Your task to perform on an android device: open app "The Home Depot" (install if not already installed) Image 0: 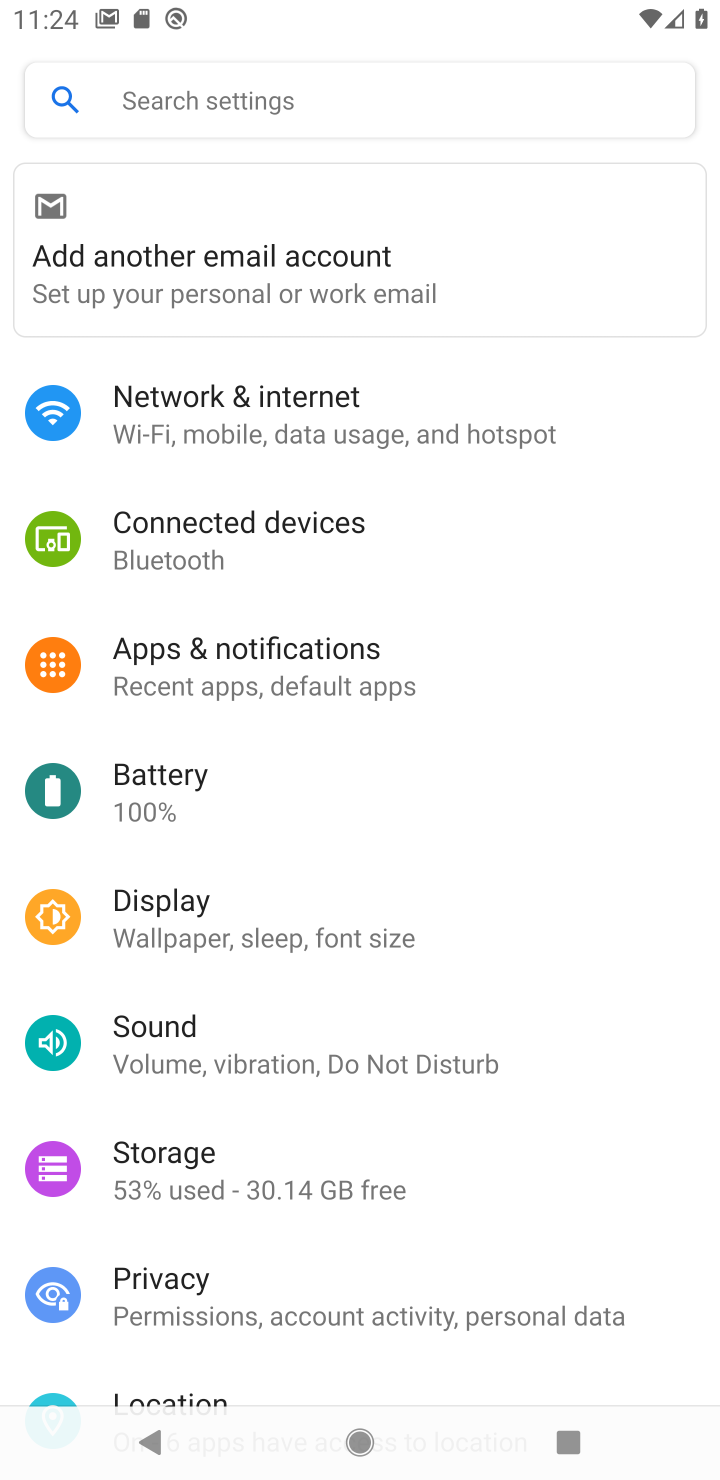
Step 0: press back button
Your task to perform on an android device: open app "The Home Depot" (install if not already installed) Image 1: 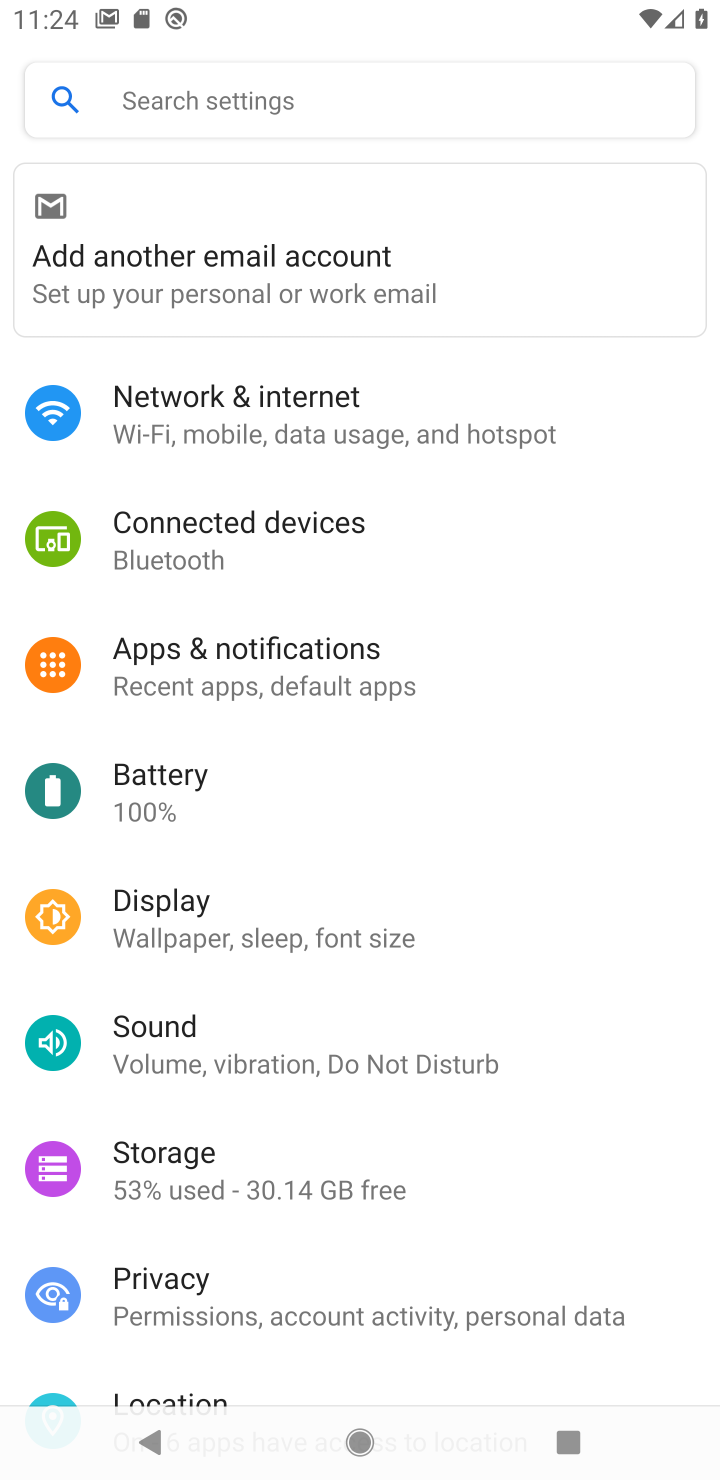
Step 1: press back button
Your task to perform on an android device: open app "The Home Depot" (install if not already installed) Image 2: 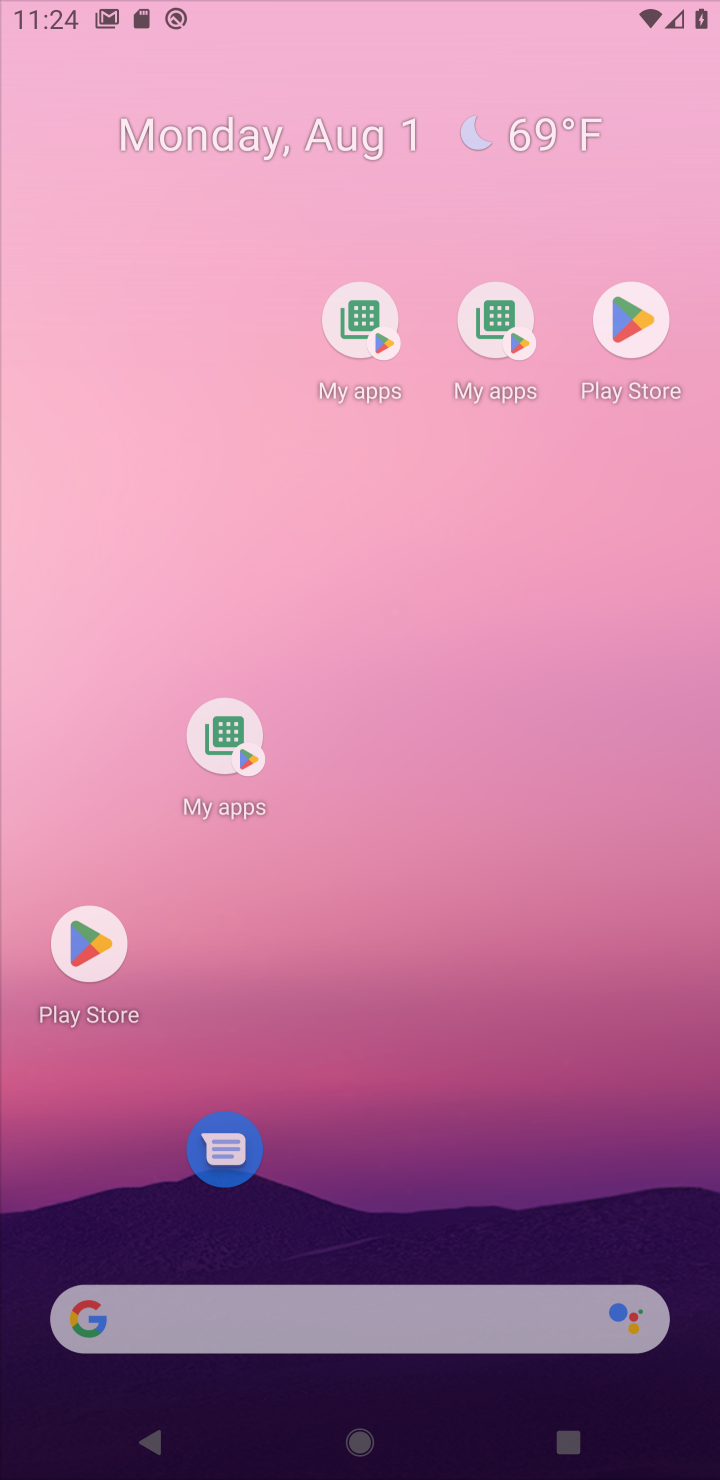
Step 2: press home button
Your task to perform on an android device: open app "The Home Depot" (install if not already installed) Image 3: 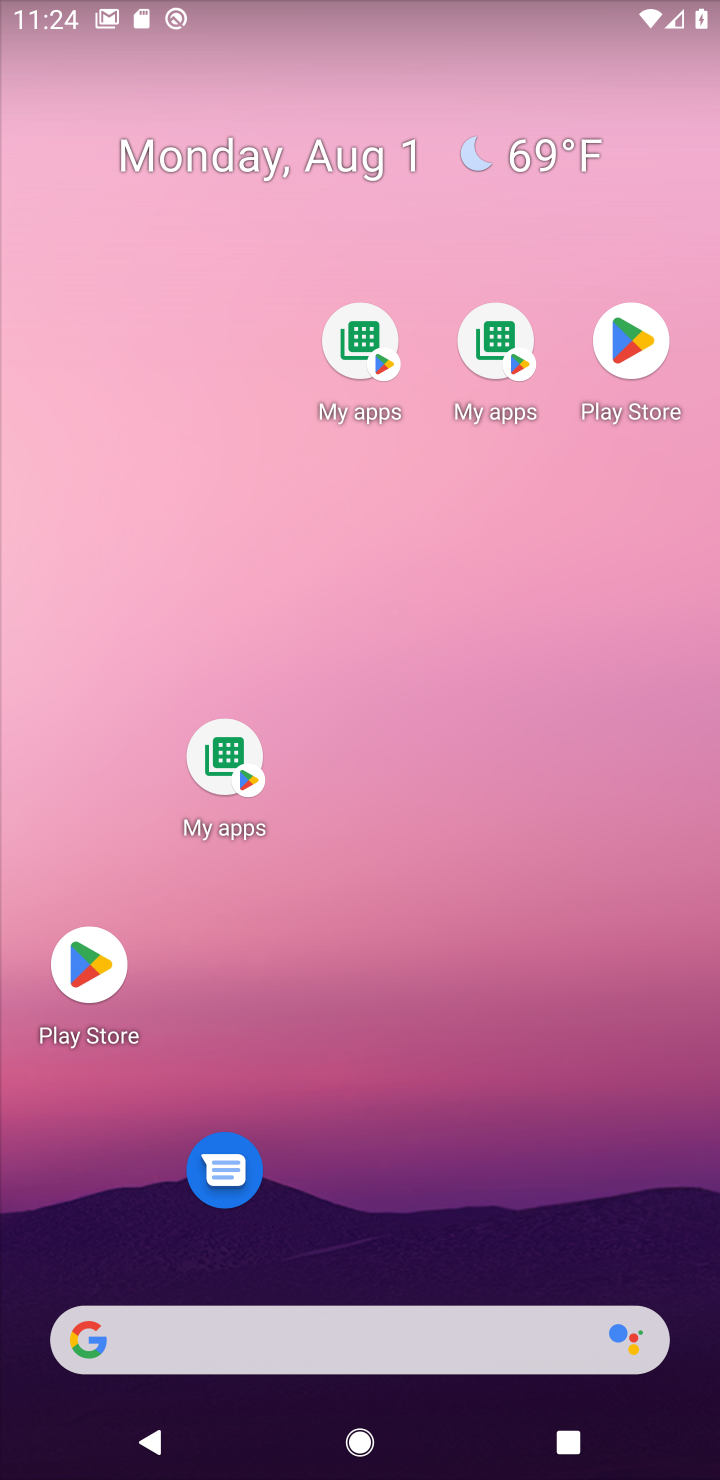
Step 3: click (639, 337)
Your task to perform on an android device: open app "The Home Depot" (install if not already installed) Image 4: 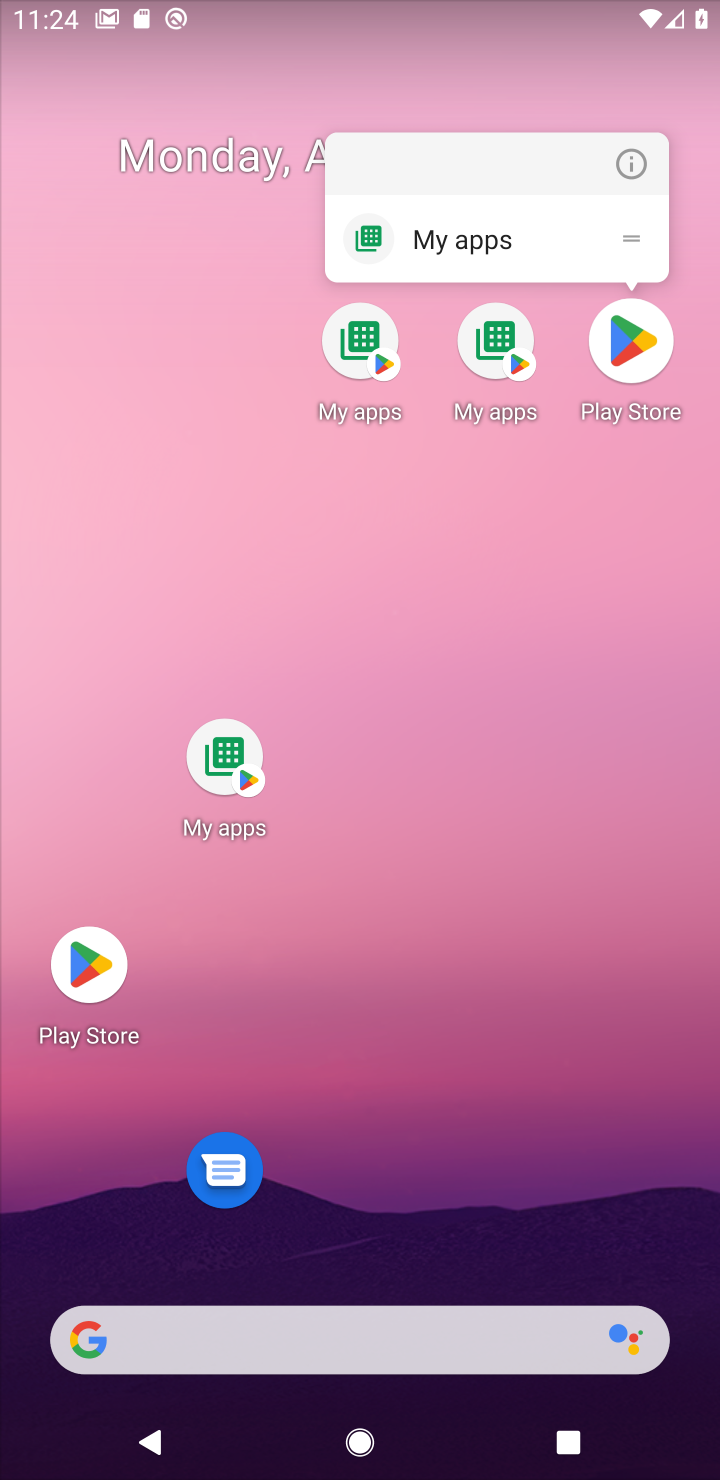
Step 4: click (639, 337)
Your task to perform on an android device: open app "The Home Depot" (install if not already installed) Image 5: 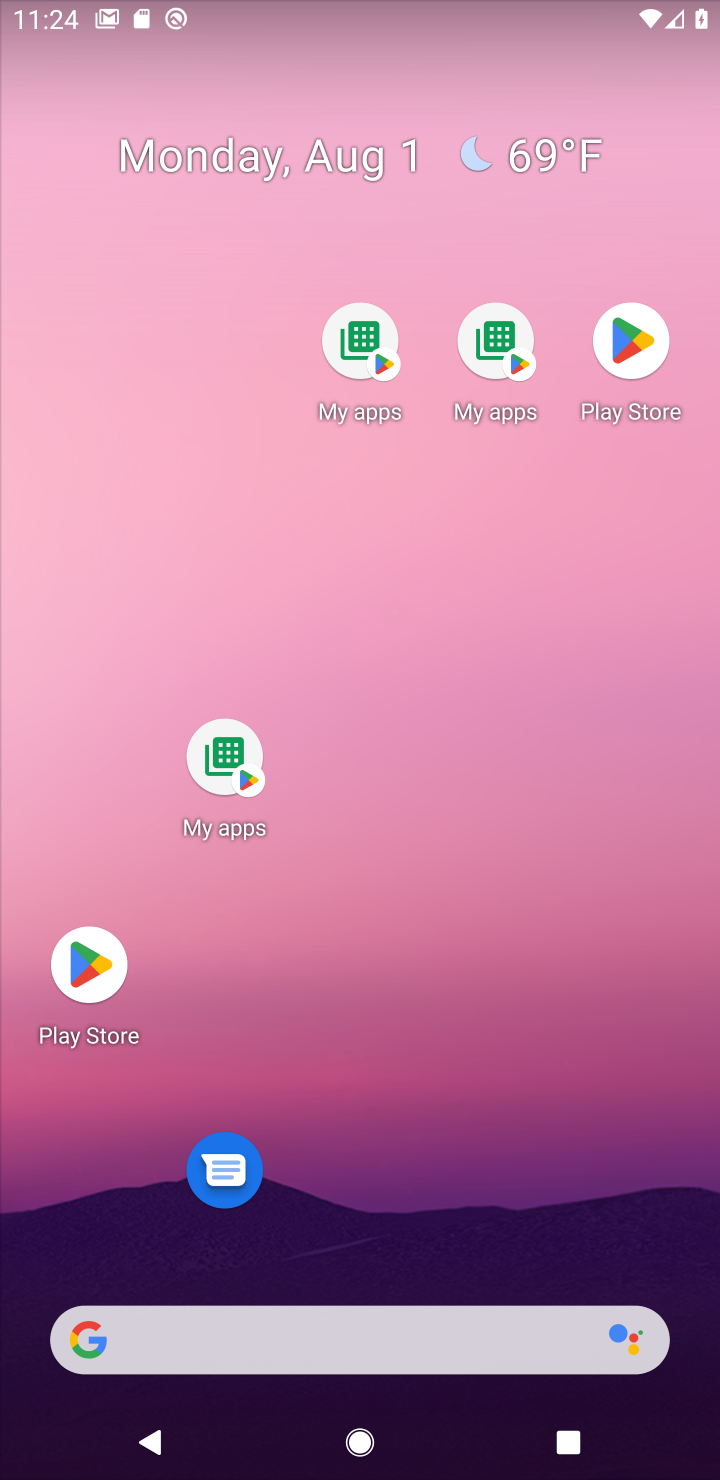
Step 5: click (439, 235)
Your task to perform on an android device: open app "The Home Depot" (install if not already installed) Image 6: 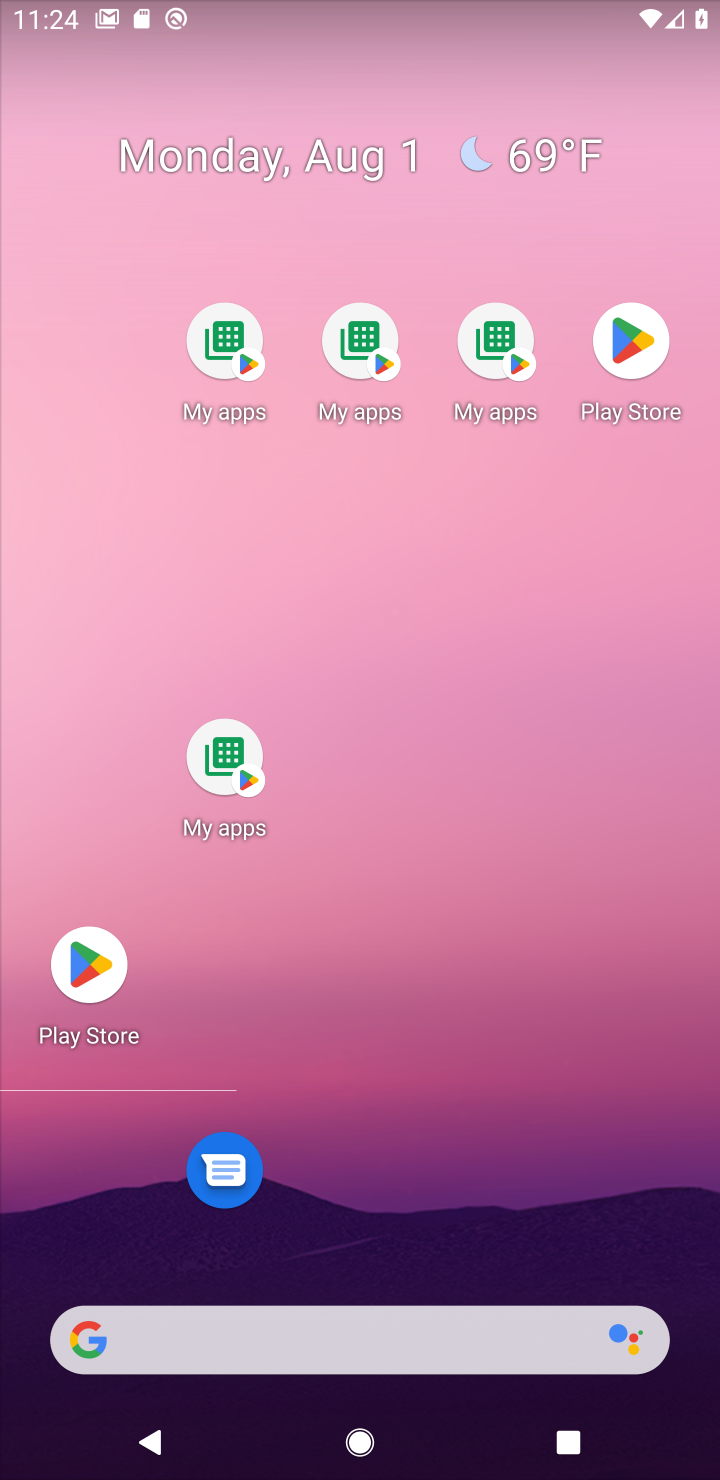
Step 6: click (474, 249)
Your task to perform on an android device: open app "The Home Depot" (install if not already installed) Image 7: 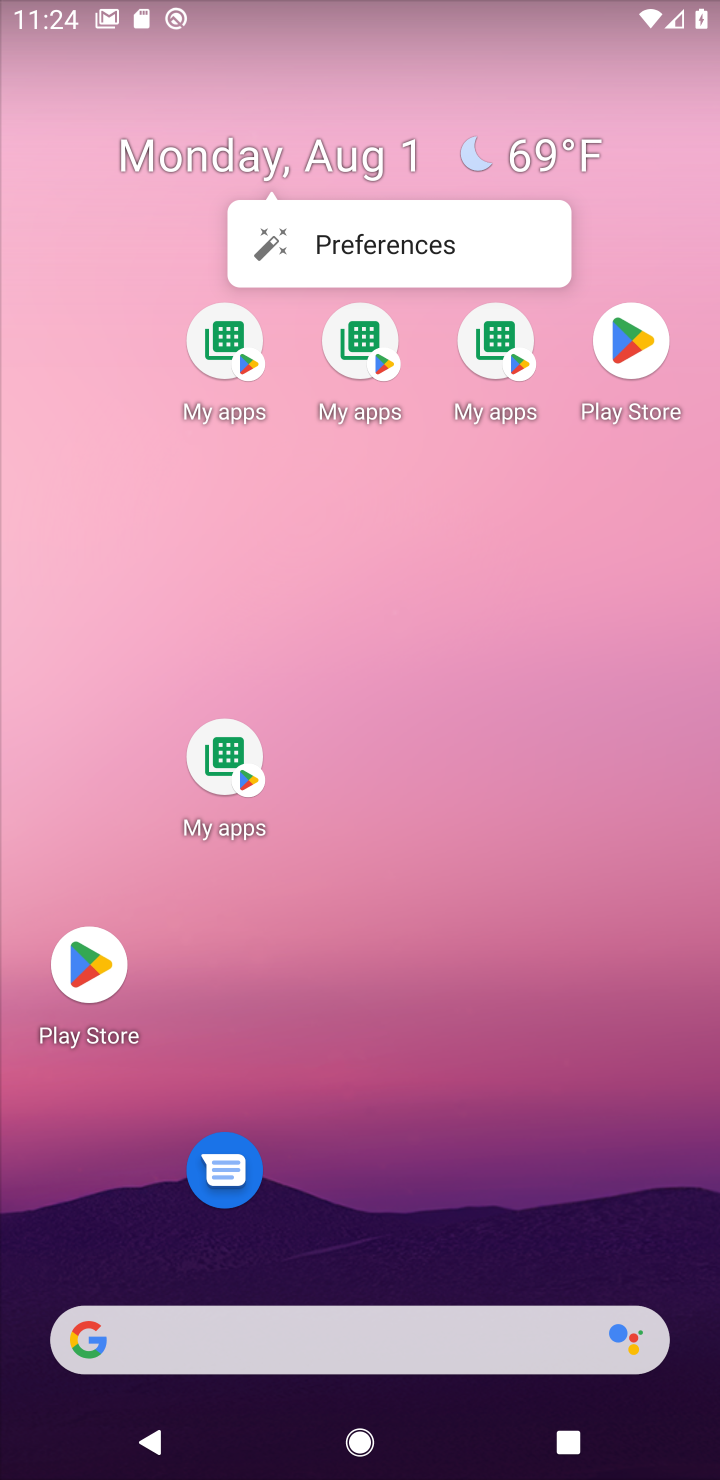
Step 7: click (636, 340)
Your task to perform on an android device: open app "The Home Depot" (install if not already installed) Image 8: 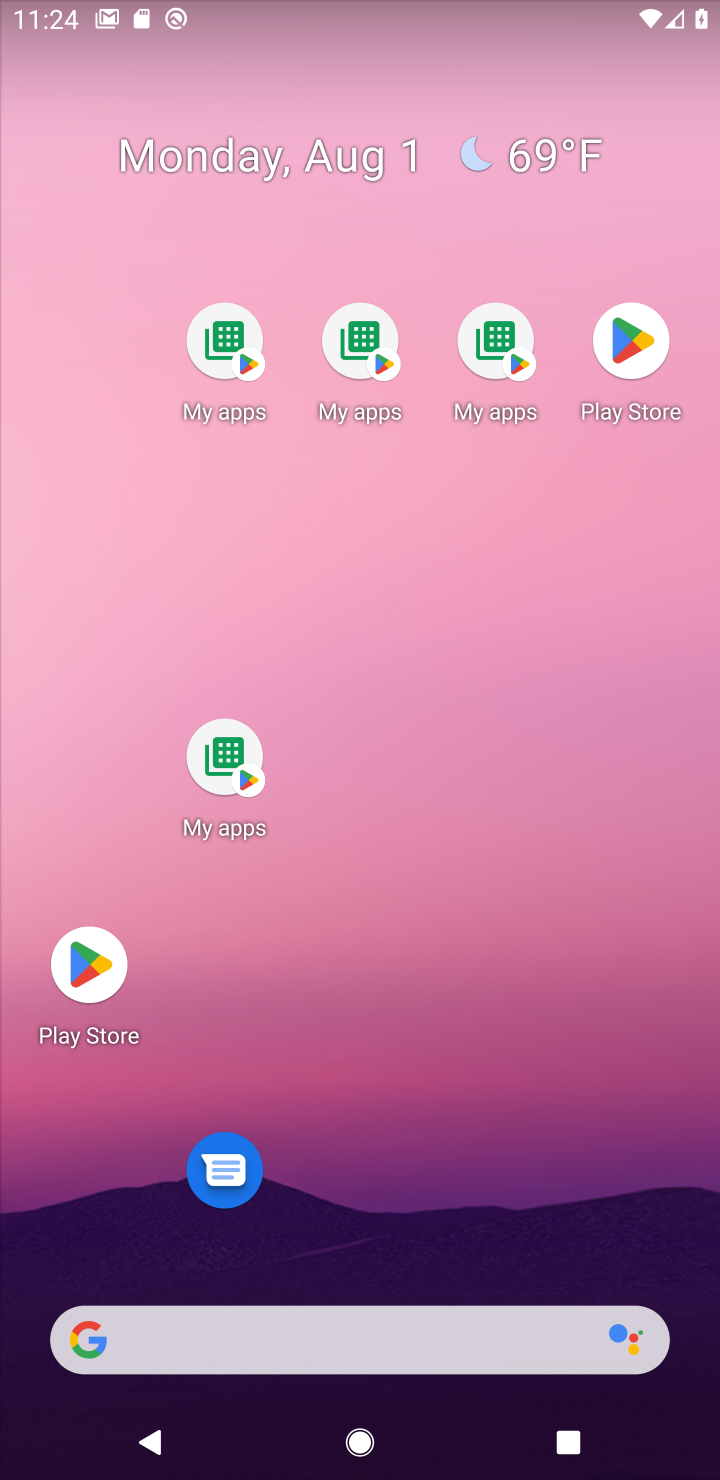
Step 8: click (614, 317)
Your task to perform on an android device: open app "The Home Depot" (install if not already installed) Image 9: 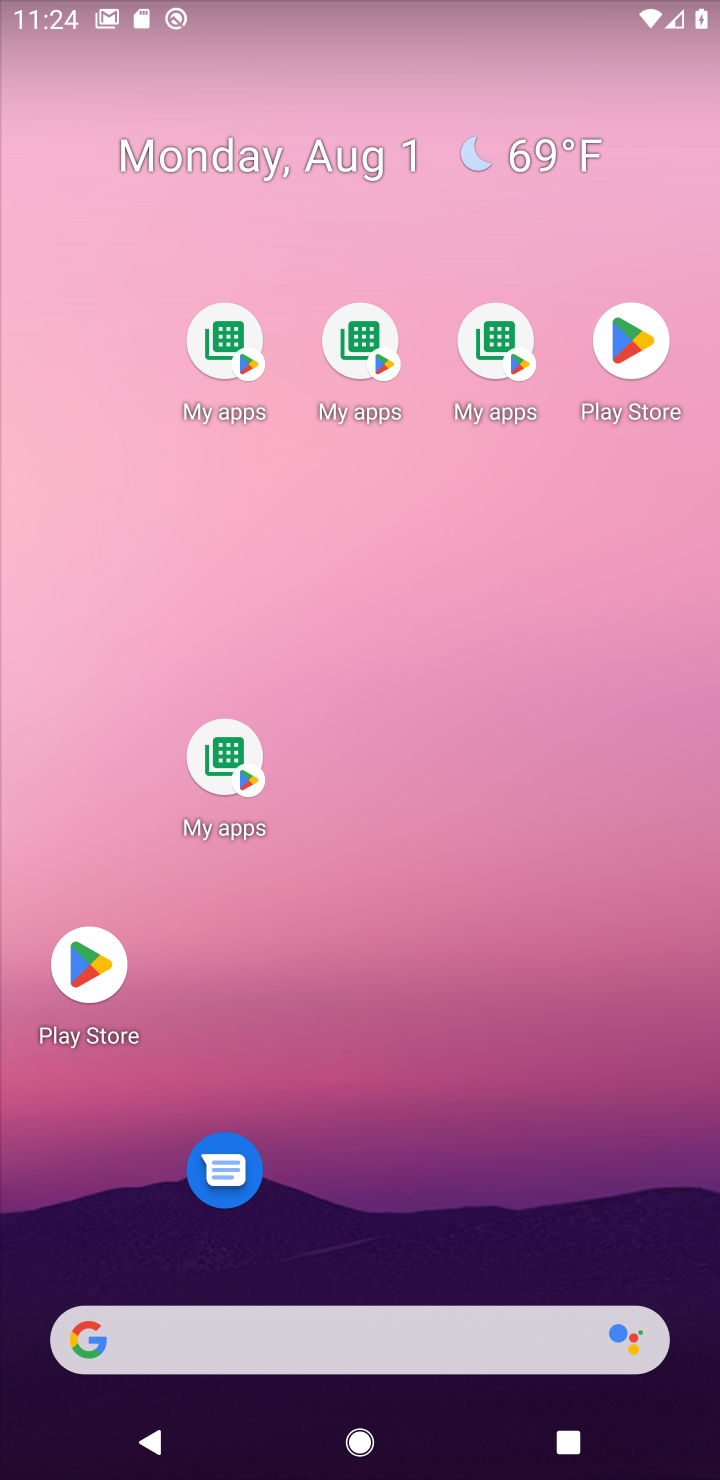
Step 9: click (613, 323)
Your task to perform on an android device: open app "The Home Depot" (install if not already installed) Image 10: 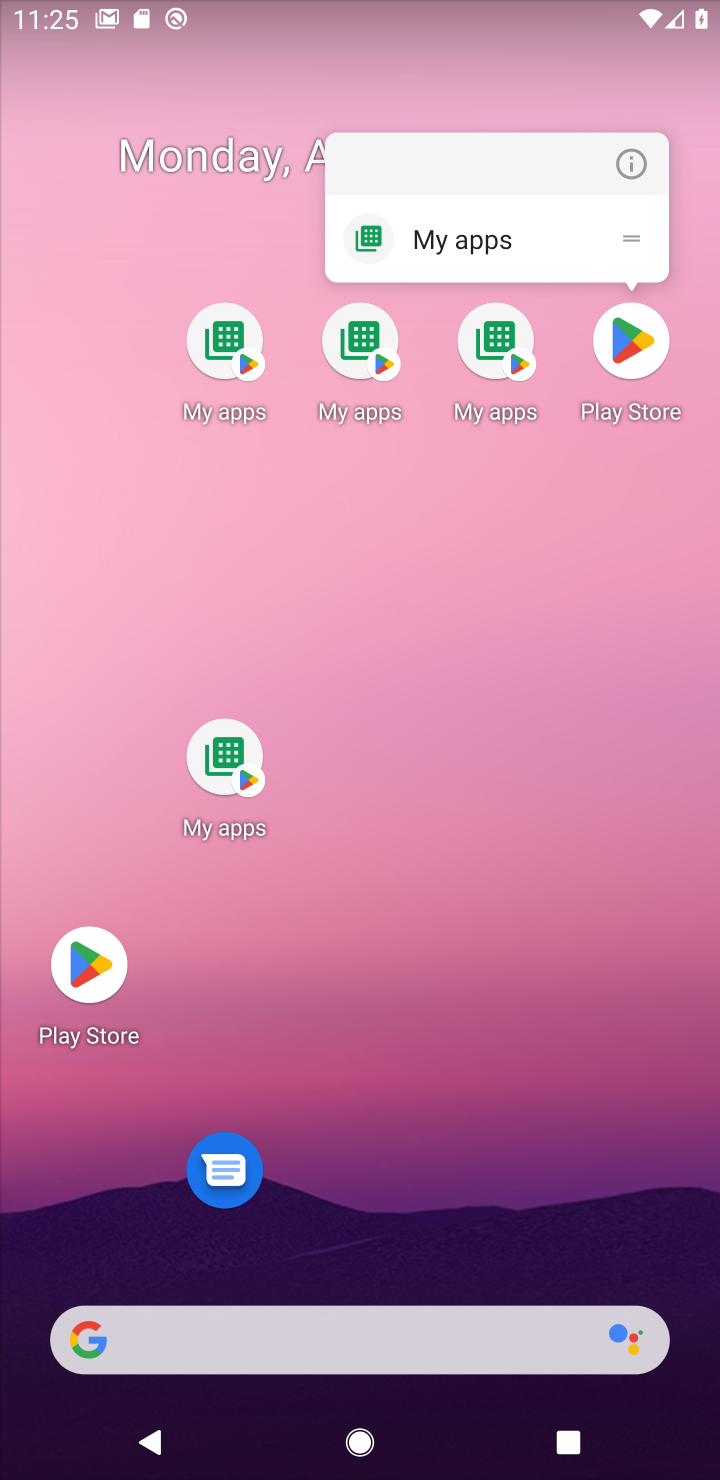
Step 10: click (386, 213)
Your task to perform on an android device: open app "The Home Depot" (install if not already installed) Image 11: 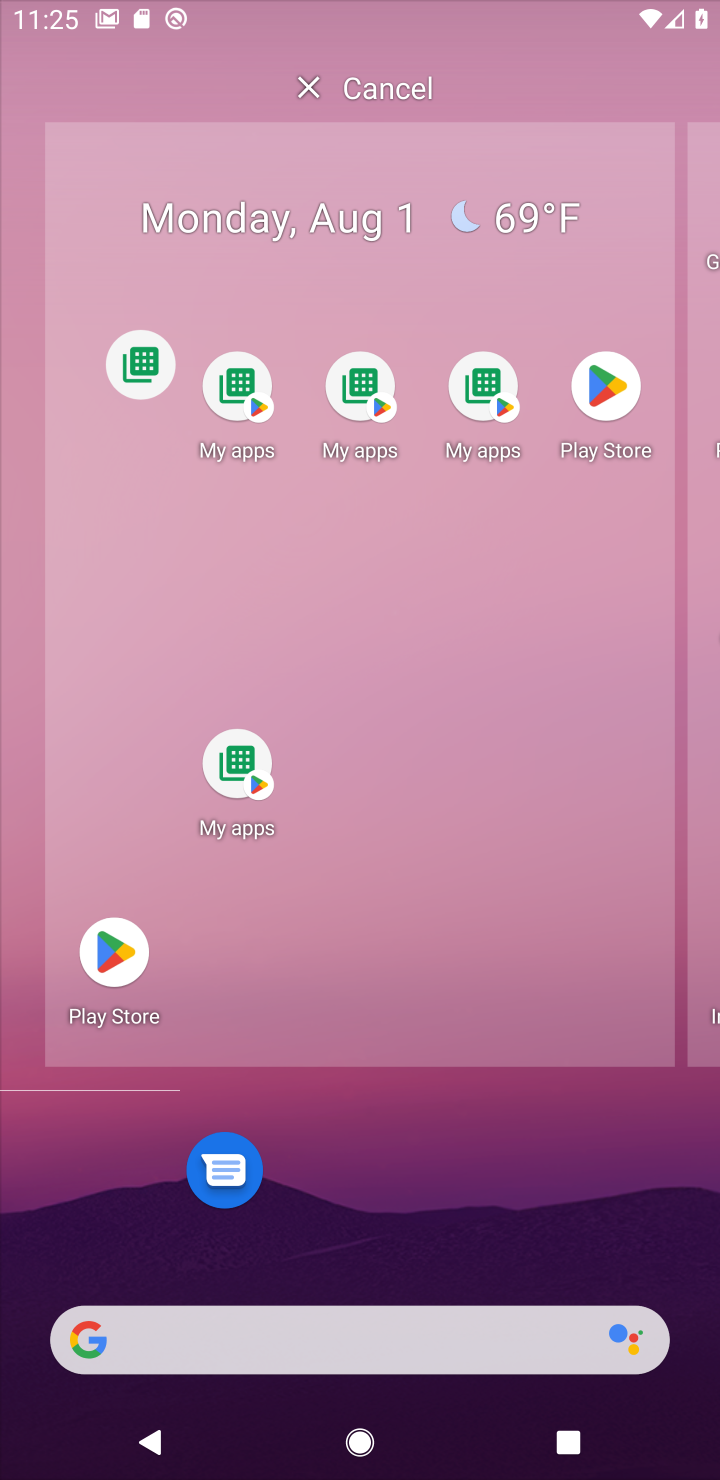
Step 11: click (488, 253)
Your task to perform on an android device: open app "The Home Depot" (install if not already installed) Image 12: 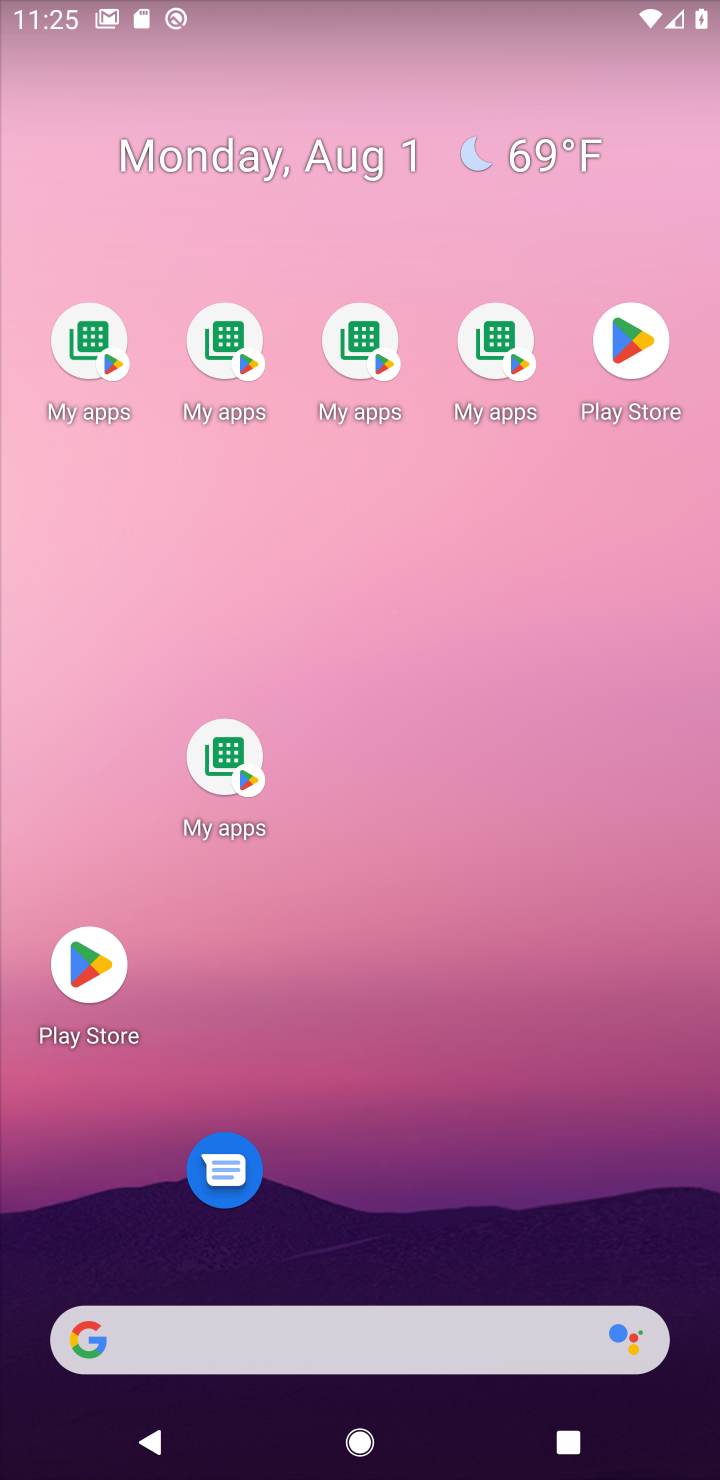
Step 12: drag from (350, 145) to (454, 337)
Your task to perform on an android device: open app "The Home Depot" (install if not already installed) Image 13: 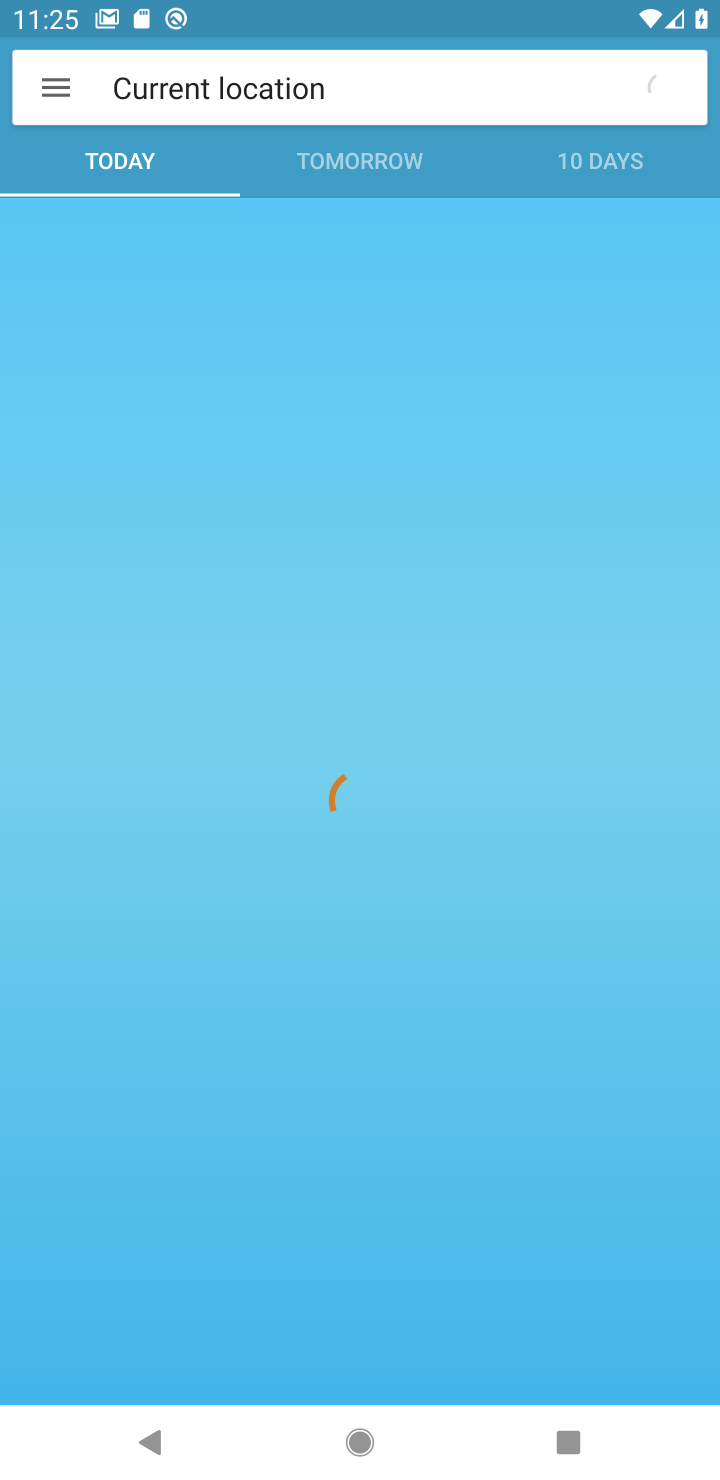
Step 13: drag from (146, 693) to (173, 238)
Your task to perform on an android device: open app "The Home Depot" (install if not already installed) Image 14: 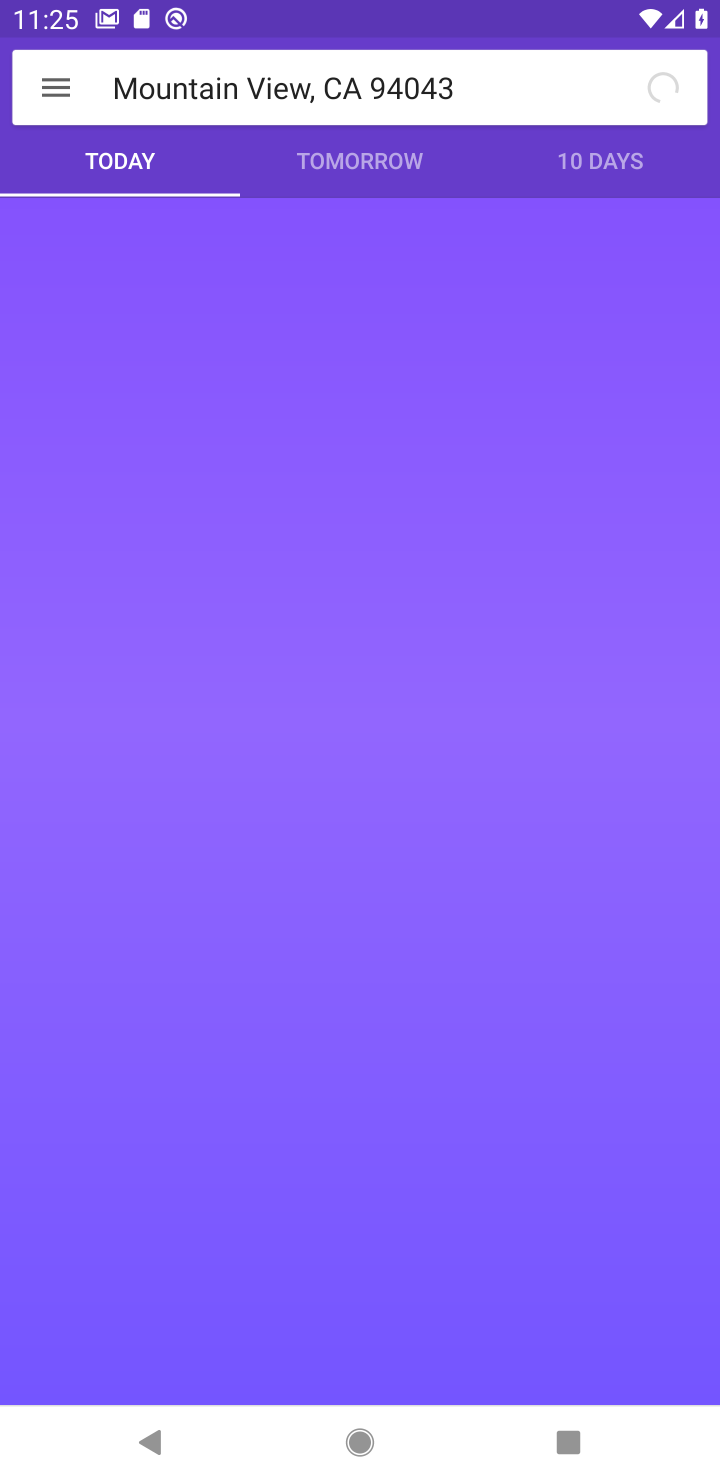
Step 14: press back button
Your task to perform on an android device: open app "The Home Depot" (install if not already installed) Image 15: 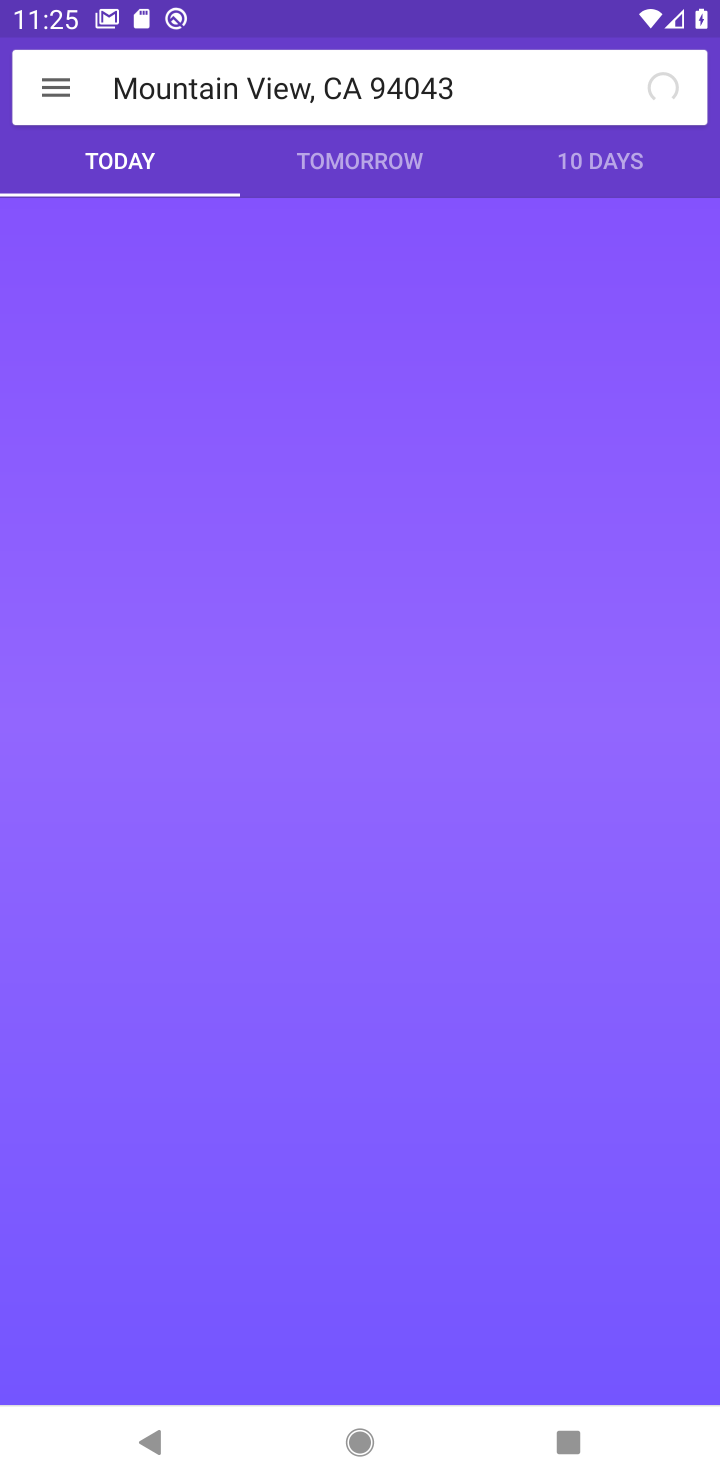
Step 15: drag from (227, 51) to (431, 190)
Your task to perform on an android device: open app "The Home Depot" (install if not already installed) Image 16: 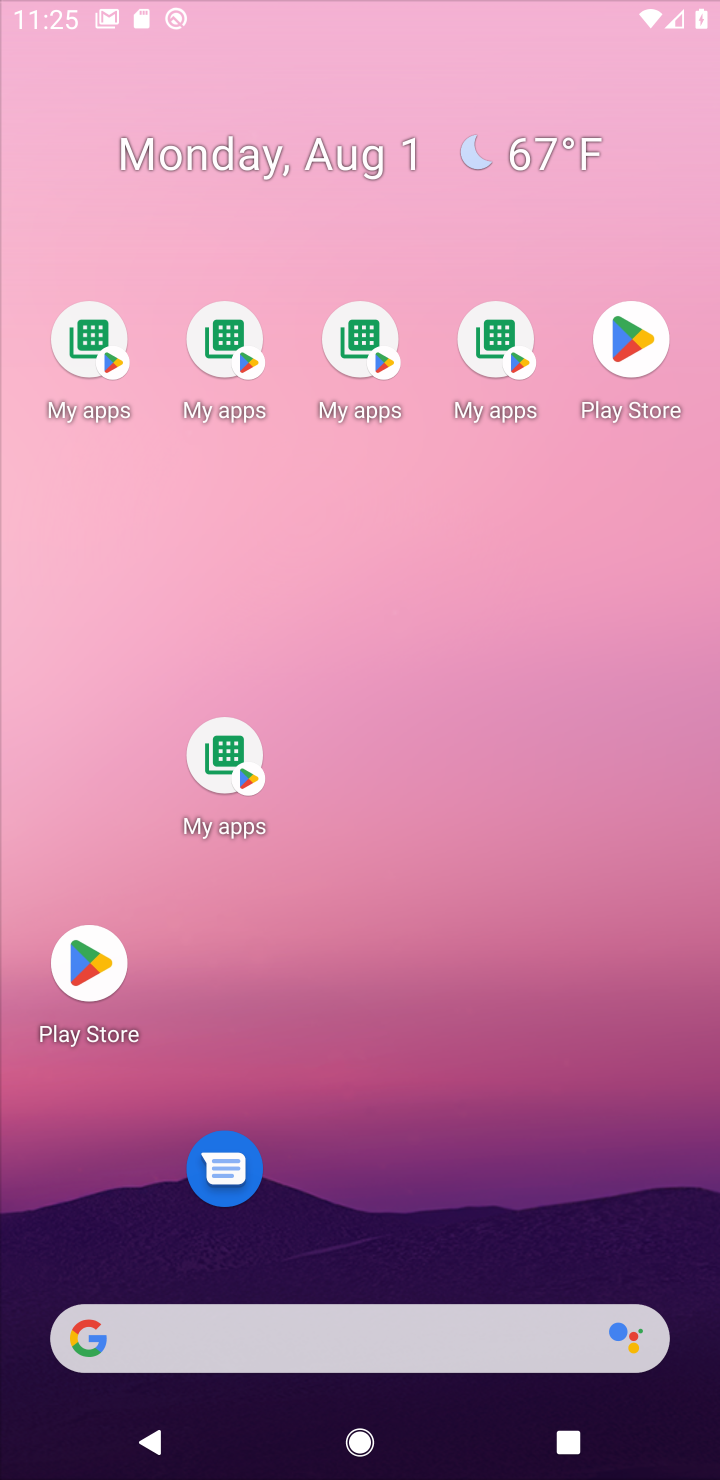
Step 16: press home button
Your task to perform on an android device: open app "The Home Depot" (install if not already installed) Image 17: 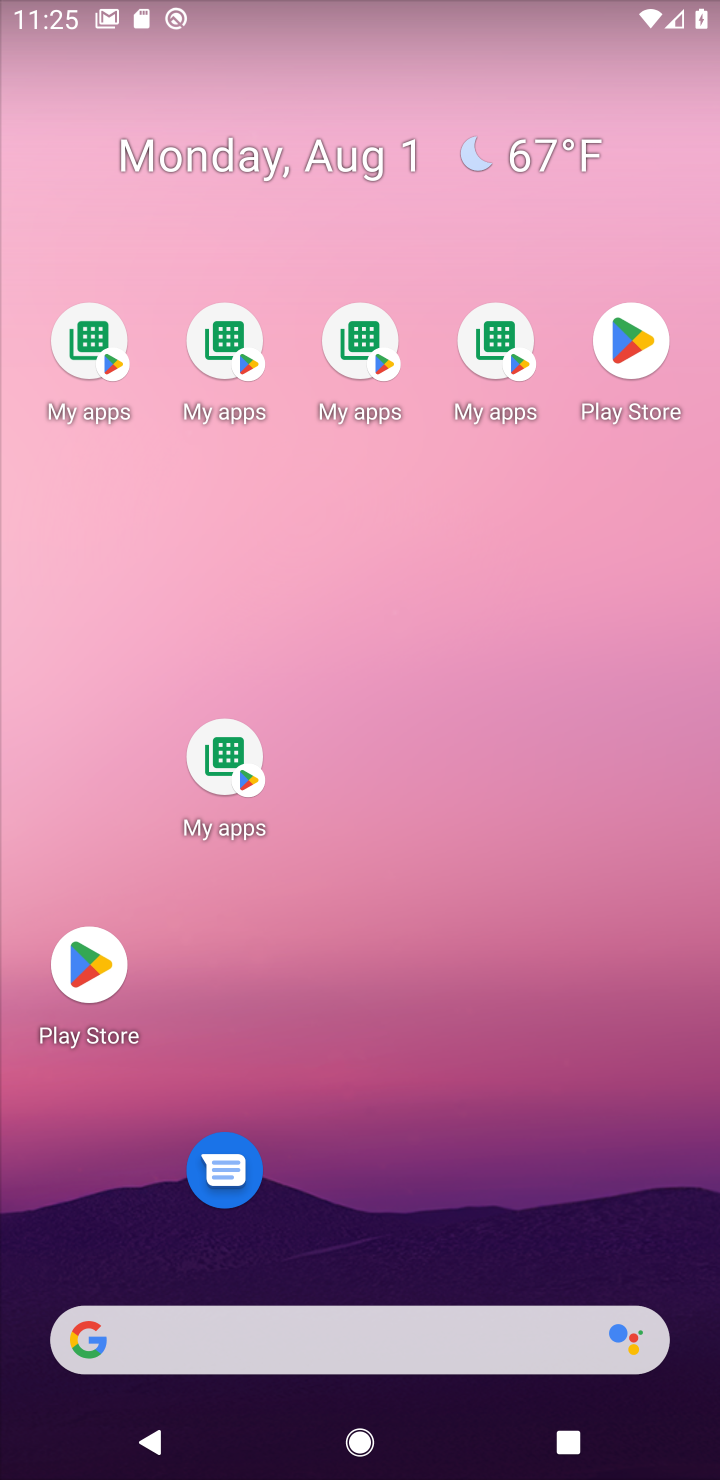
Step 17: click (360, 524)
Your task to perform on an android device: open app "The Home Depot" (install if not already installed) Image 18: 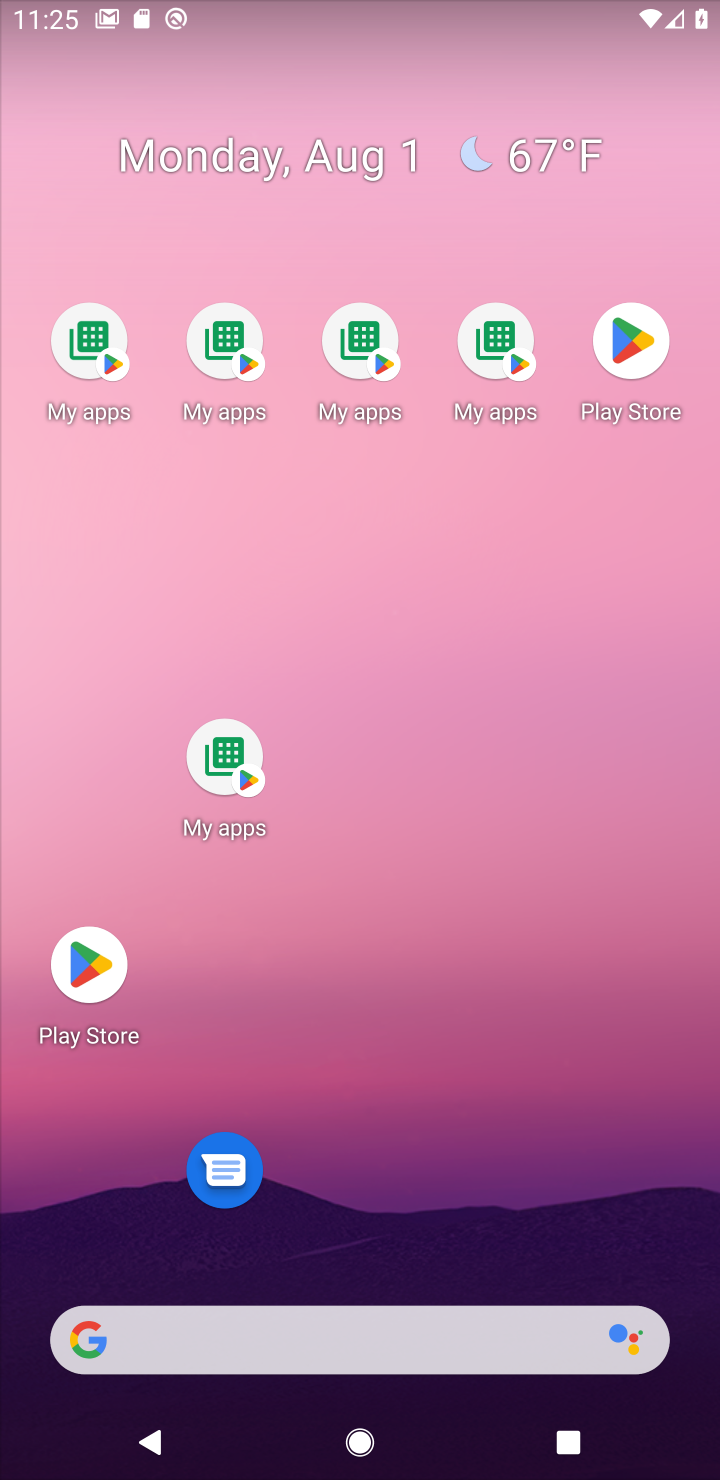
Step 18: drag from (404, 463) to (454, 138)
Your task to perform on an android device: open app "The Home Depot" (install if not already installed) Image 19: 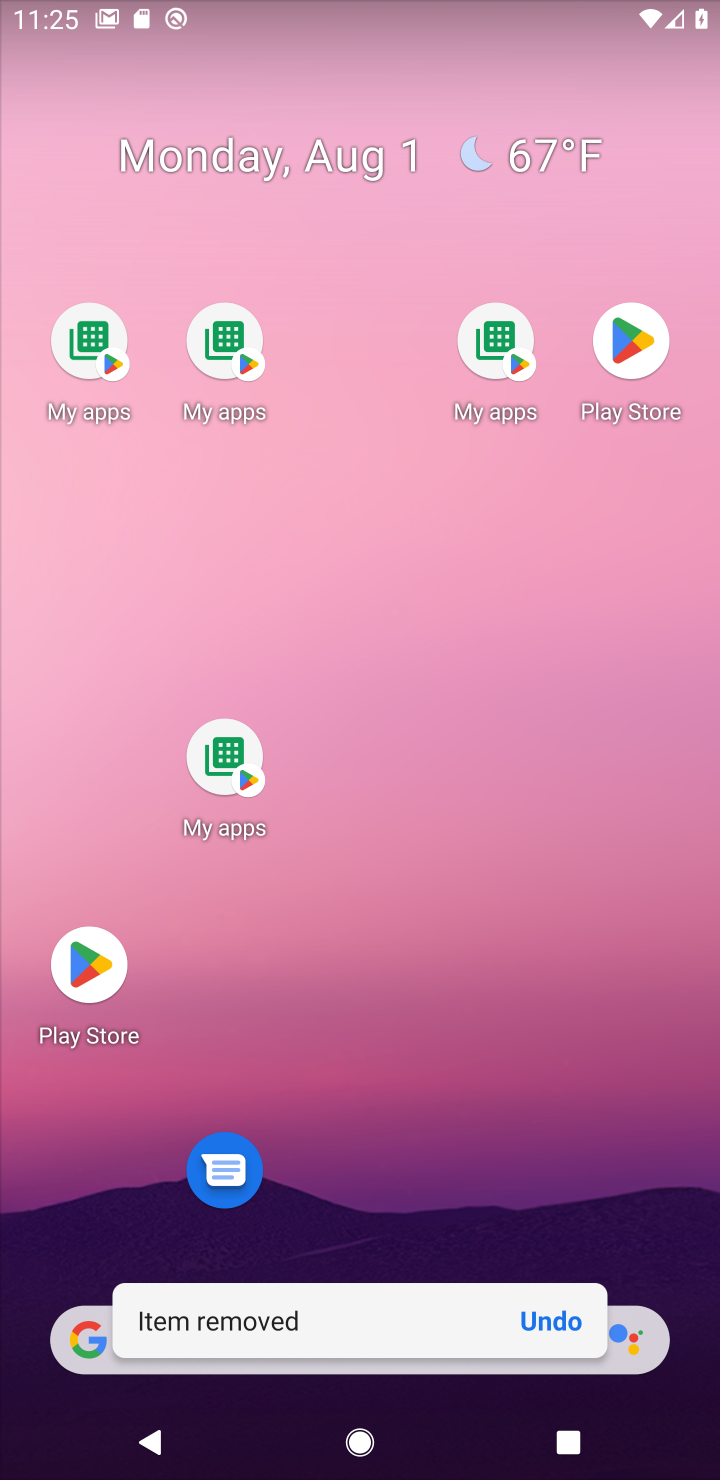
Step 19: click (79, 960)
Your task to perform on an android device: open app "The Home Depot" (install if not already installed) Image 20: 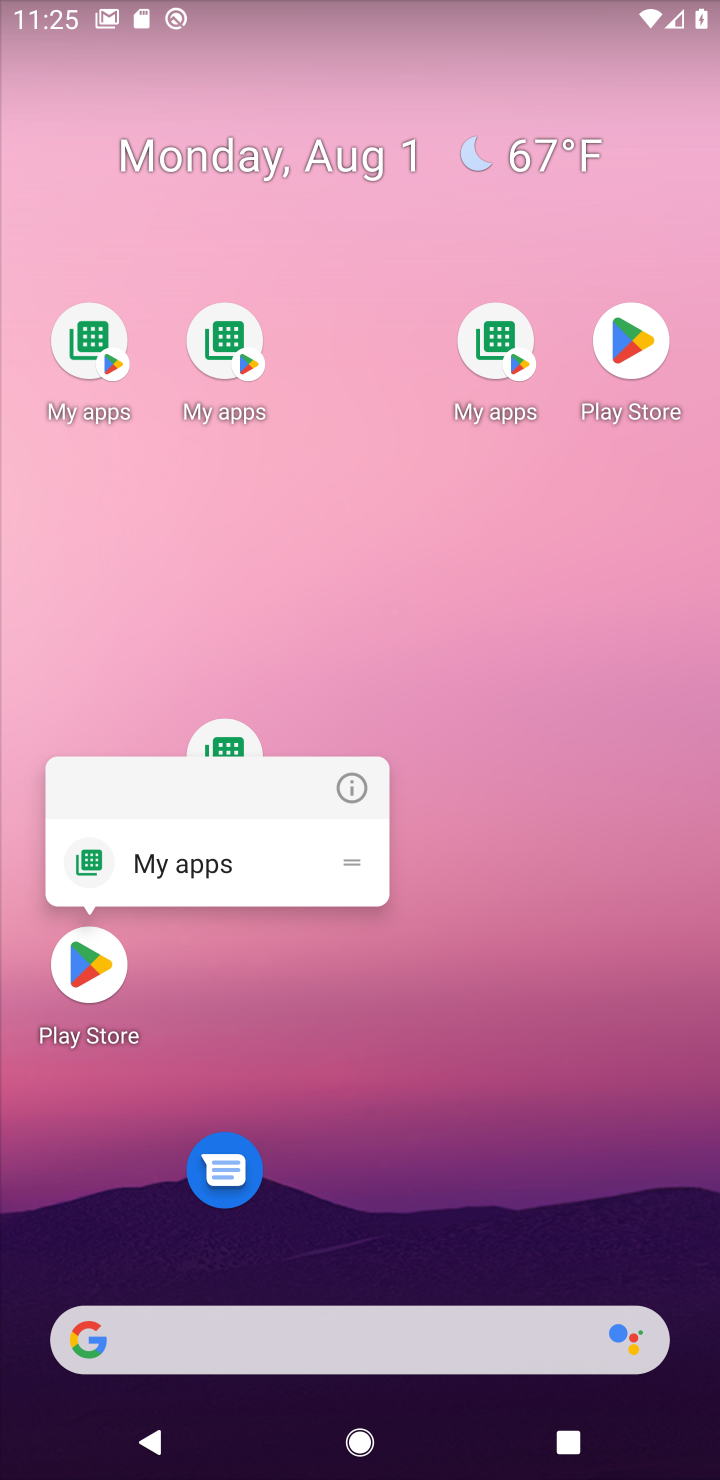
Step 20: click (111, 982)
Your task to perform on an android device: open app "The Home Depot" (install if not already installed) Image 21: 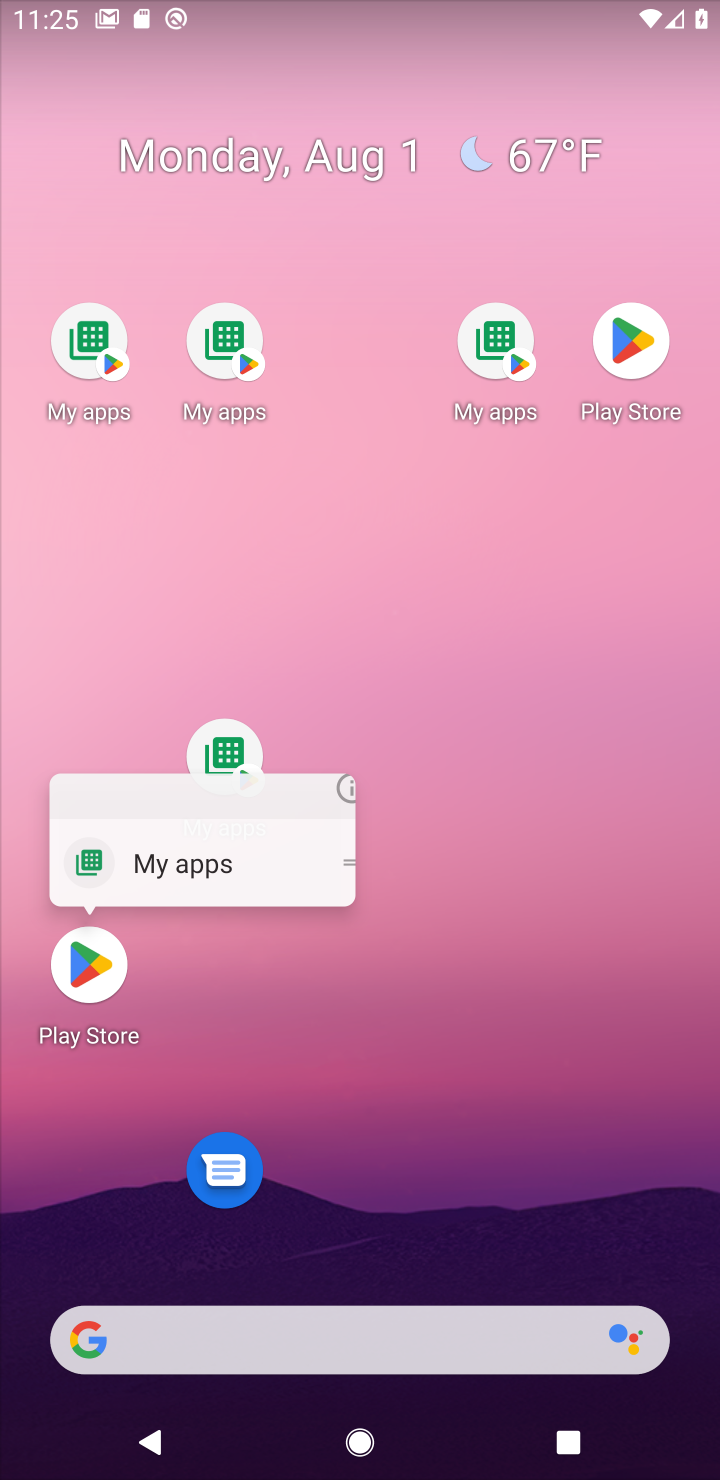
Step 21: click (104, 975)
Your task to perform on an android device: open app "The Home Depot" (install if not already installed) Image 22: 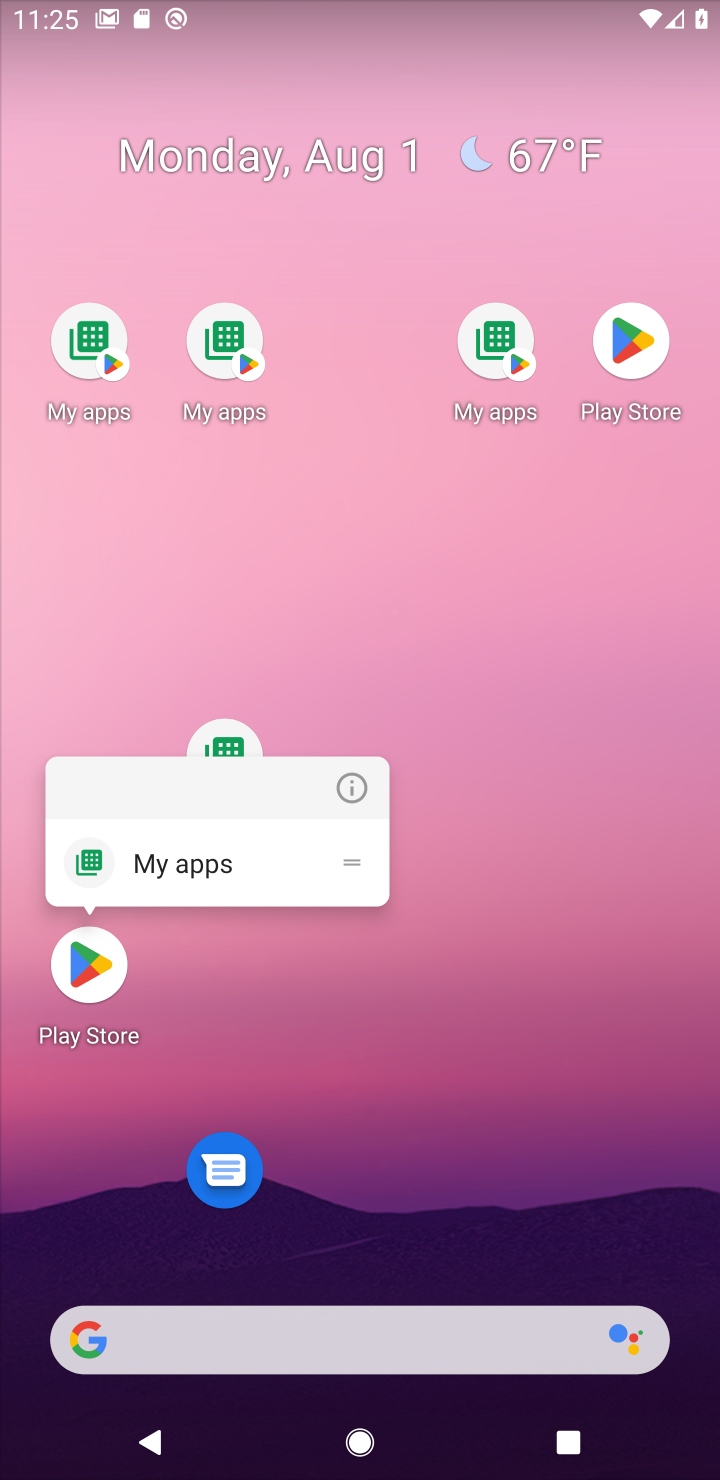
Step 22: drag from (257, 258) to (397, 26)
Your task to perform on an android device: open app "The Home Depot" (install if not already installed) Image 23: 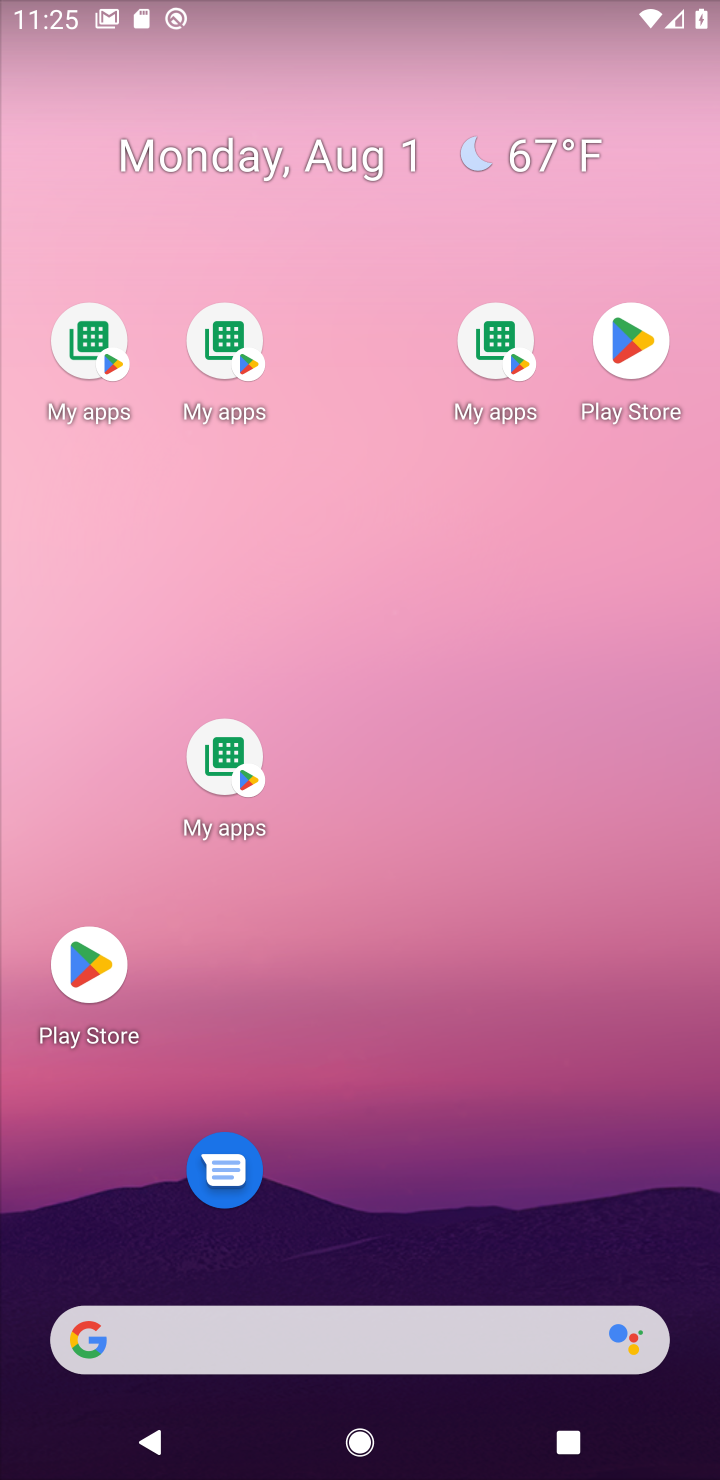
Step 23: click (441, 28)
Your task to perform on an android device: open app "The Home Depot" (install if not already installed) Image 24: 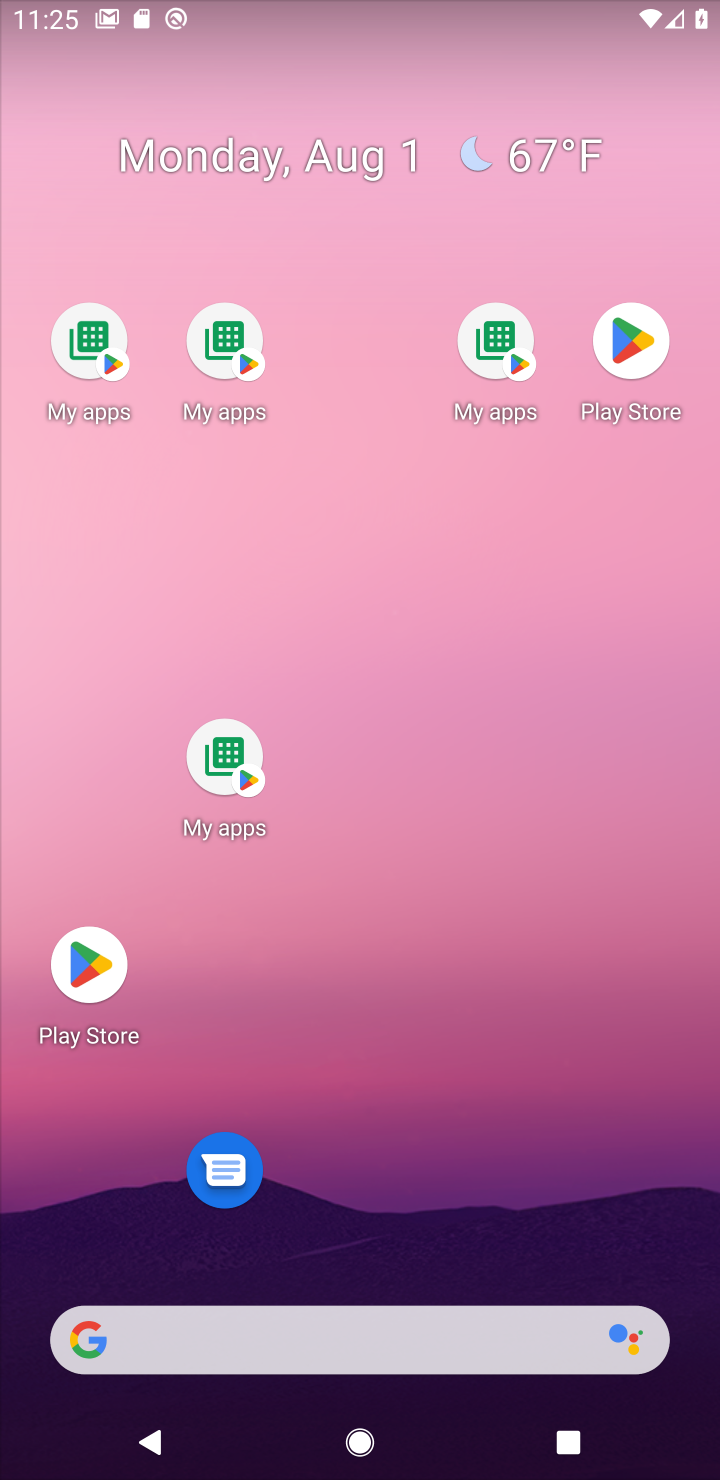
Step 24: drag from (428, 966) to (332, 230)
Your task to perform on an android device: open app "The Home Depot" (install if not already installed) Image 25: 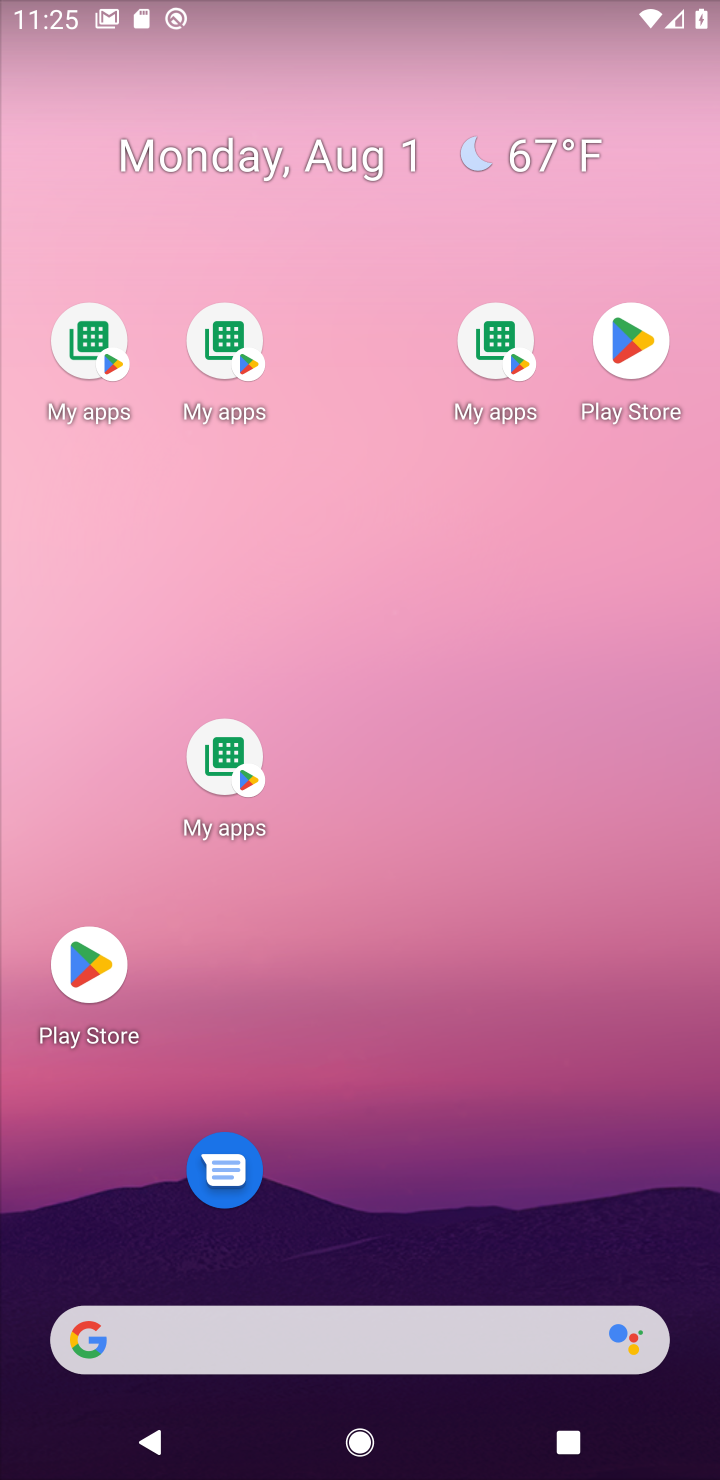
Step 25: click (617, 330)
Your task to perform on an android device: open app "The Home Depot" (install if not already installed) Image 26: 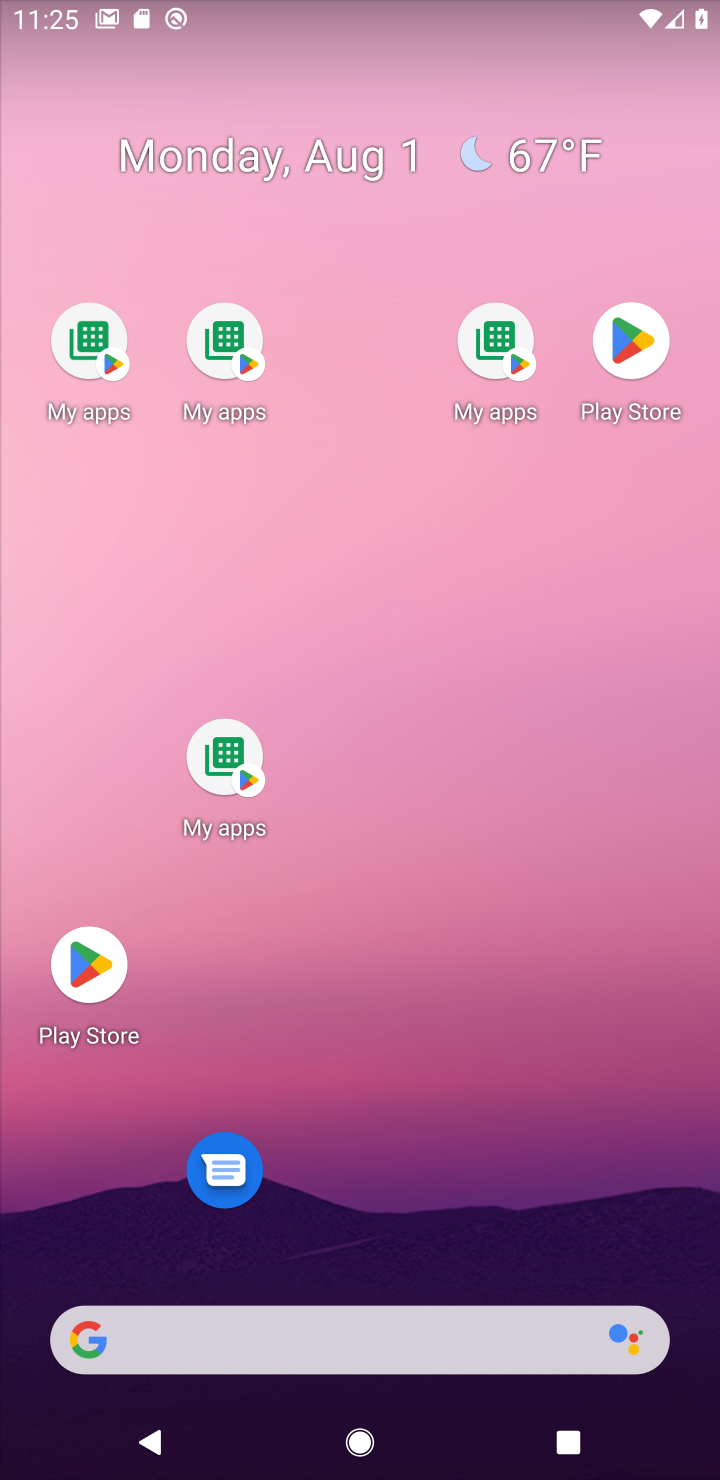
Step 26: click (613, 346)
Your task to perform on an android device: open app "The Home Depot" (install if not already installed) Image 27: 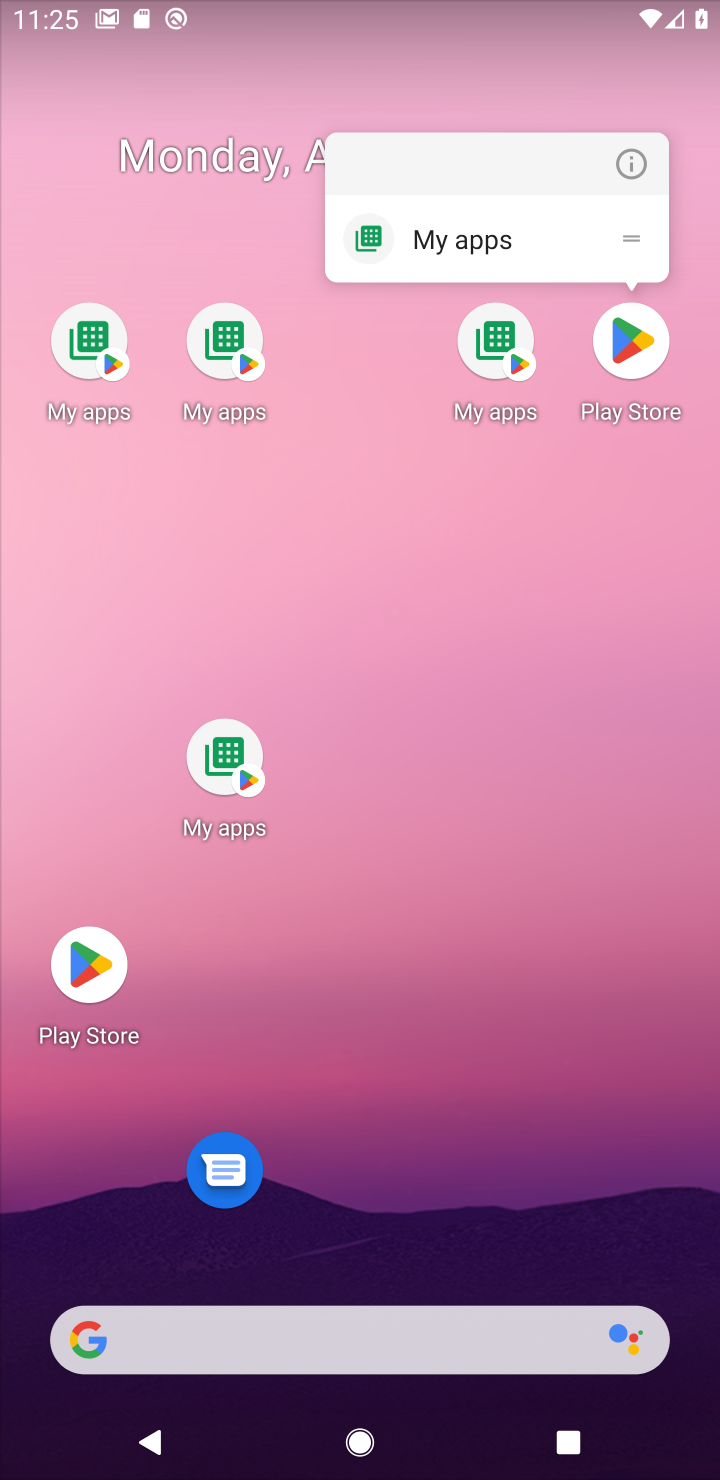
Step 27: click (634, 340)
Your task to perform on an android device: open app "The Home Depot" (install if not already installed) Image 28: 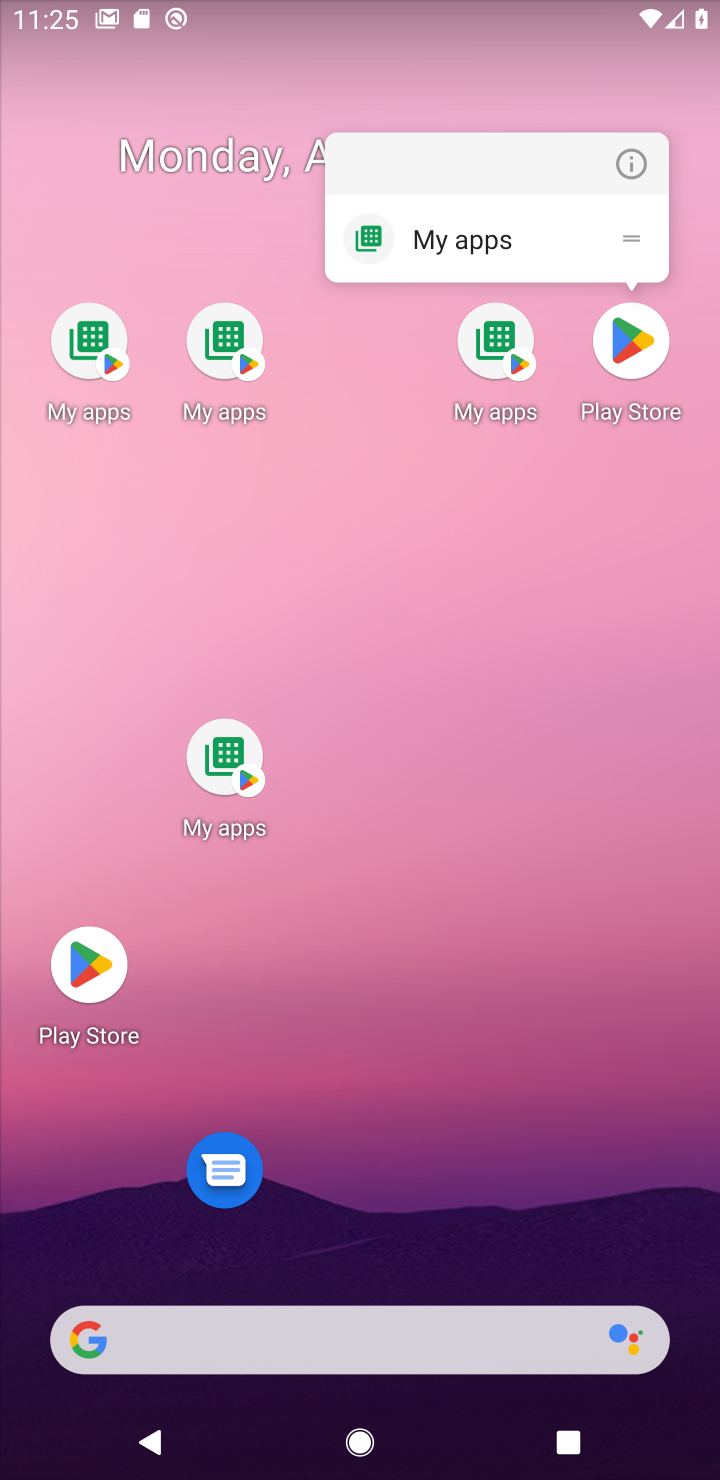
Step 28: click (632, 347)
Your task to perform on an android device: open app "The Home Depot" (install if not already installed) Image 29: 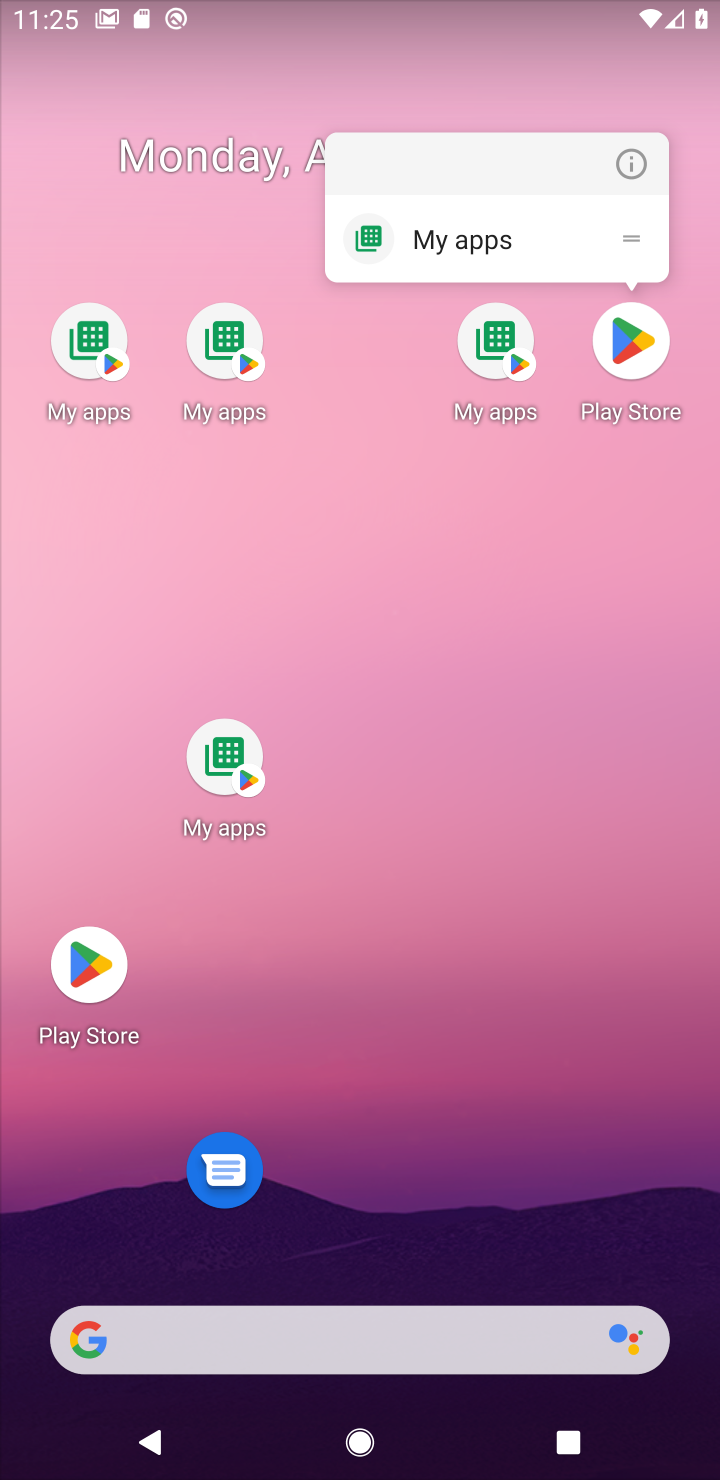
Step 29: click (630, 349)
Your task to perform on an android device: open app "The Home Depot" (install if not already installed) Image 30: 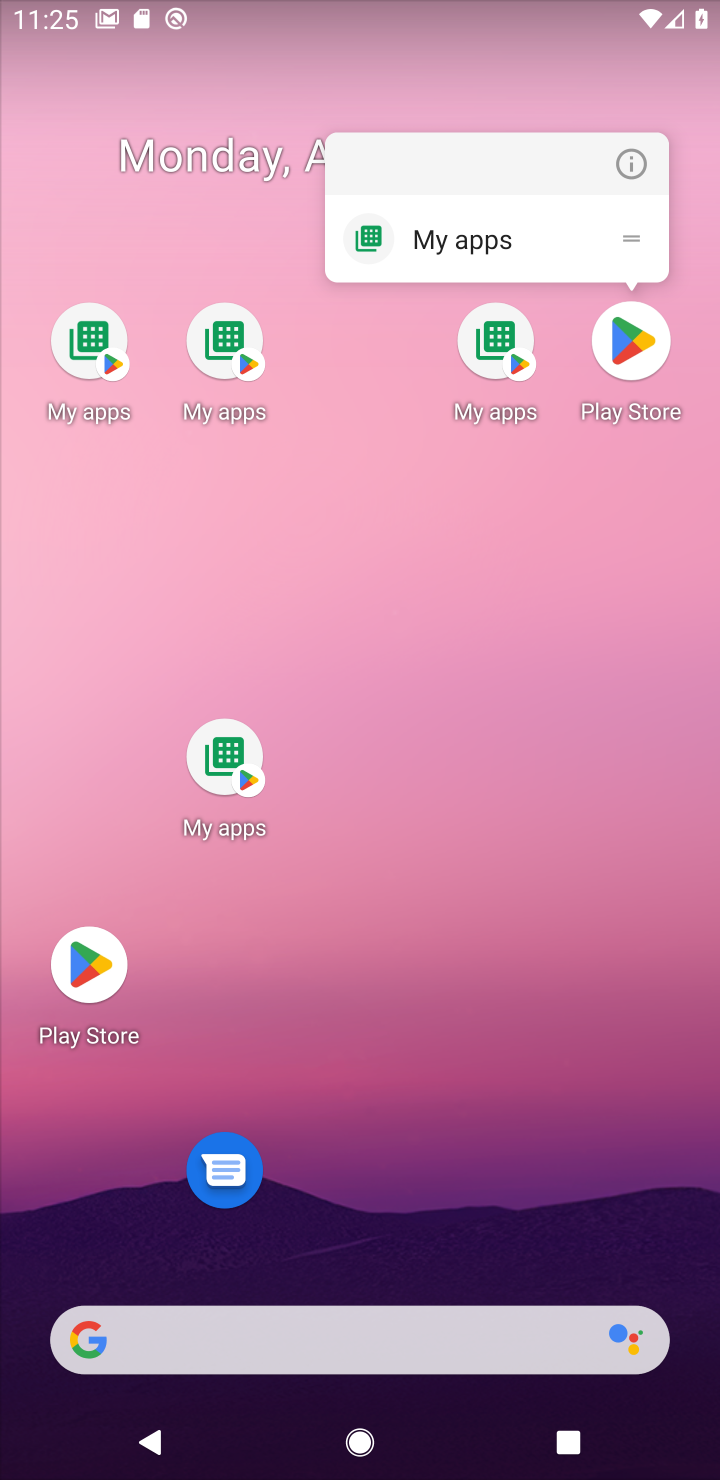
Step 30: click (614, 343)
Your task to perform on an android device: open app "The Home Depot" (install if not already installed) Image 31: 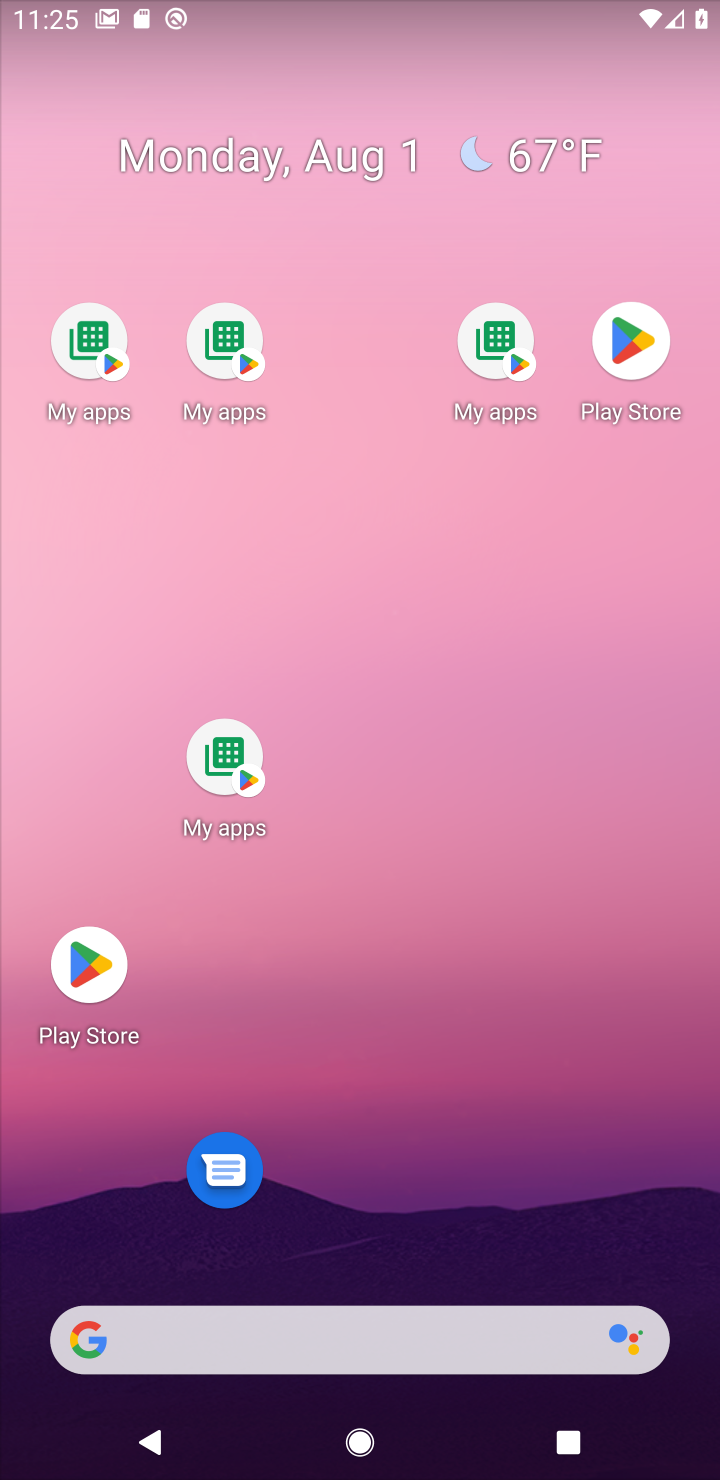
Step 31: click (618, 338)
Your task to perform on an android device: open app "The Home Depot" (install if not already installed) Image 32: 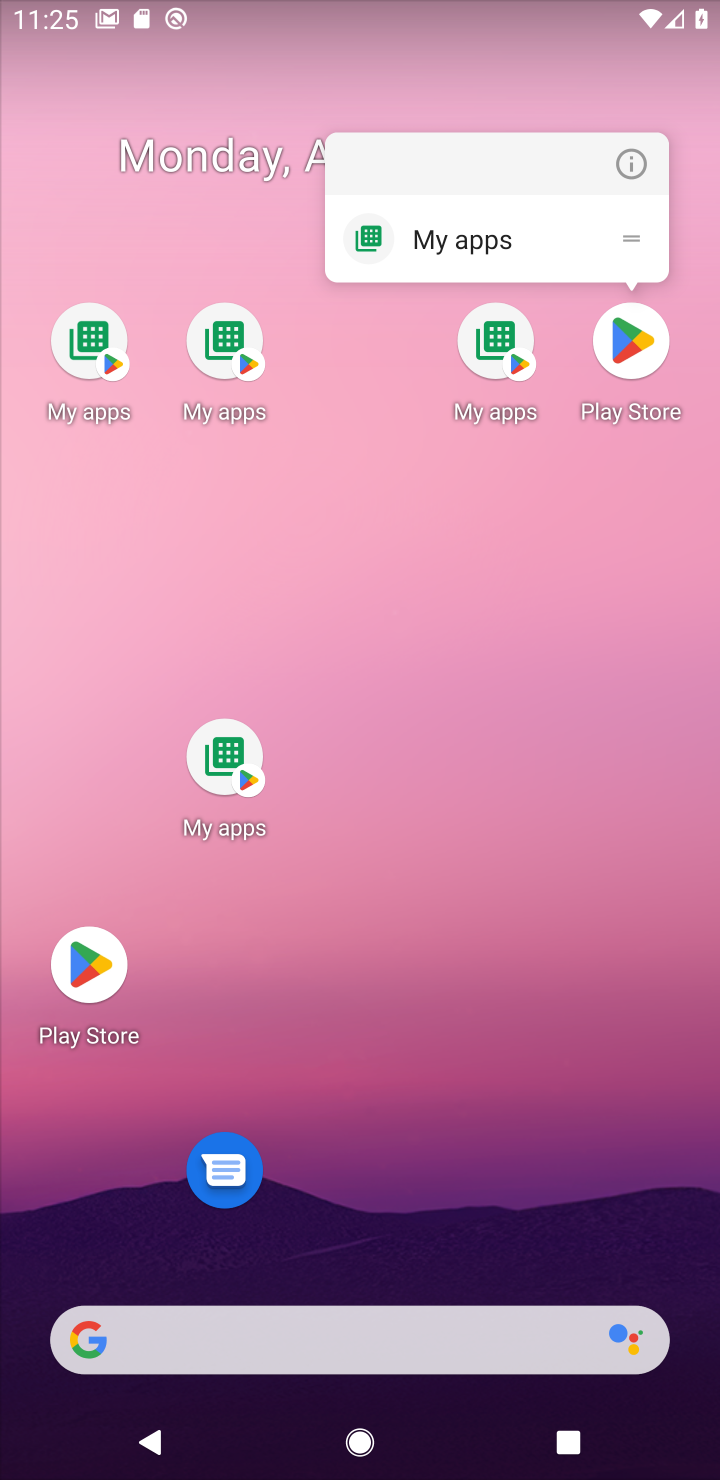
Step 32: click (632, 350)
Your task to perform on an android device: open app "The Home Depot" (install if not already installed) Image 33: 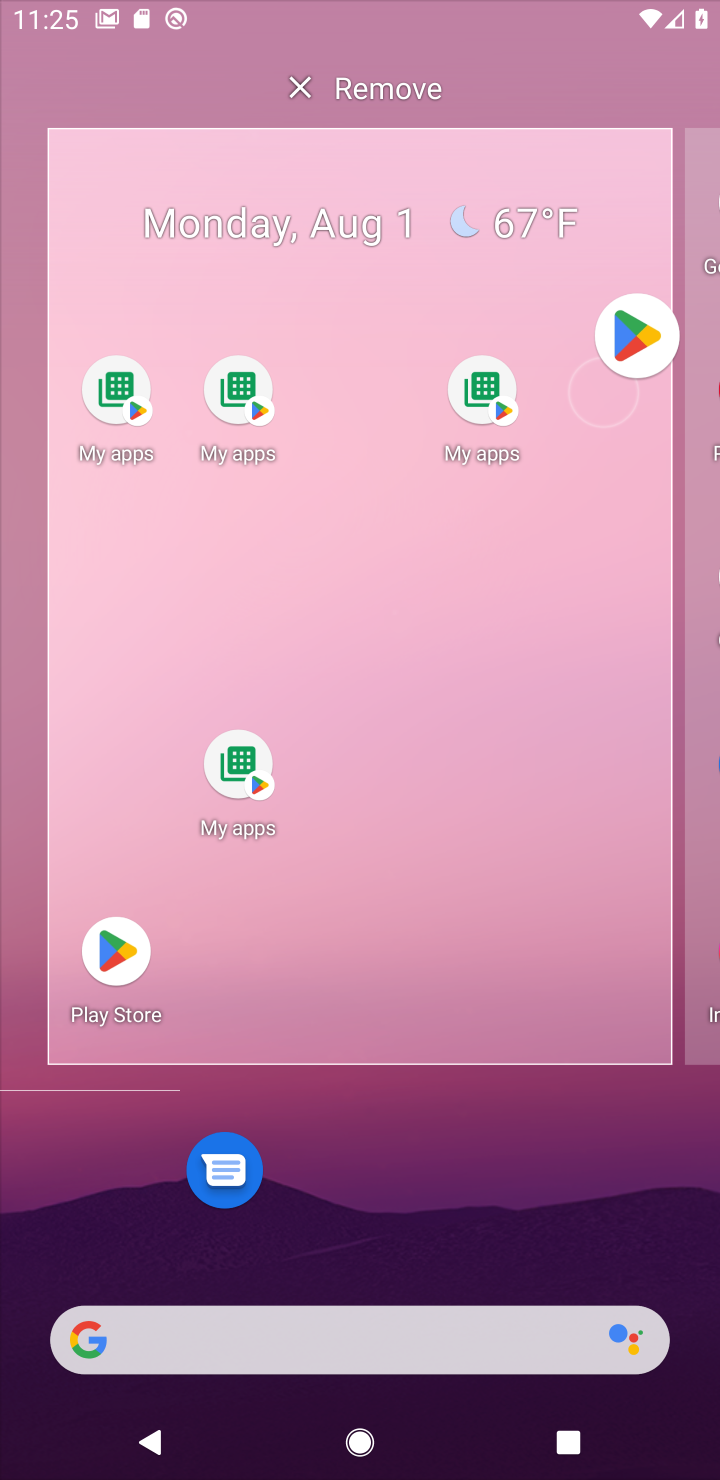
Step 33: click (659, 338)
Your task to perform on an android device: open app "The Home Depot" (install if not already installed) Image 34: 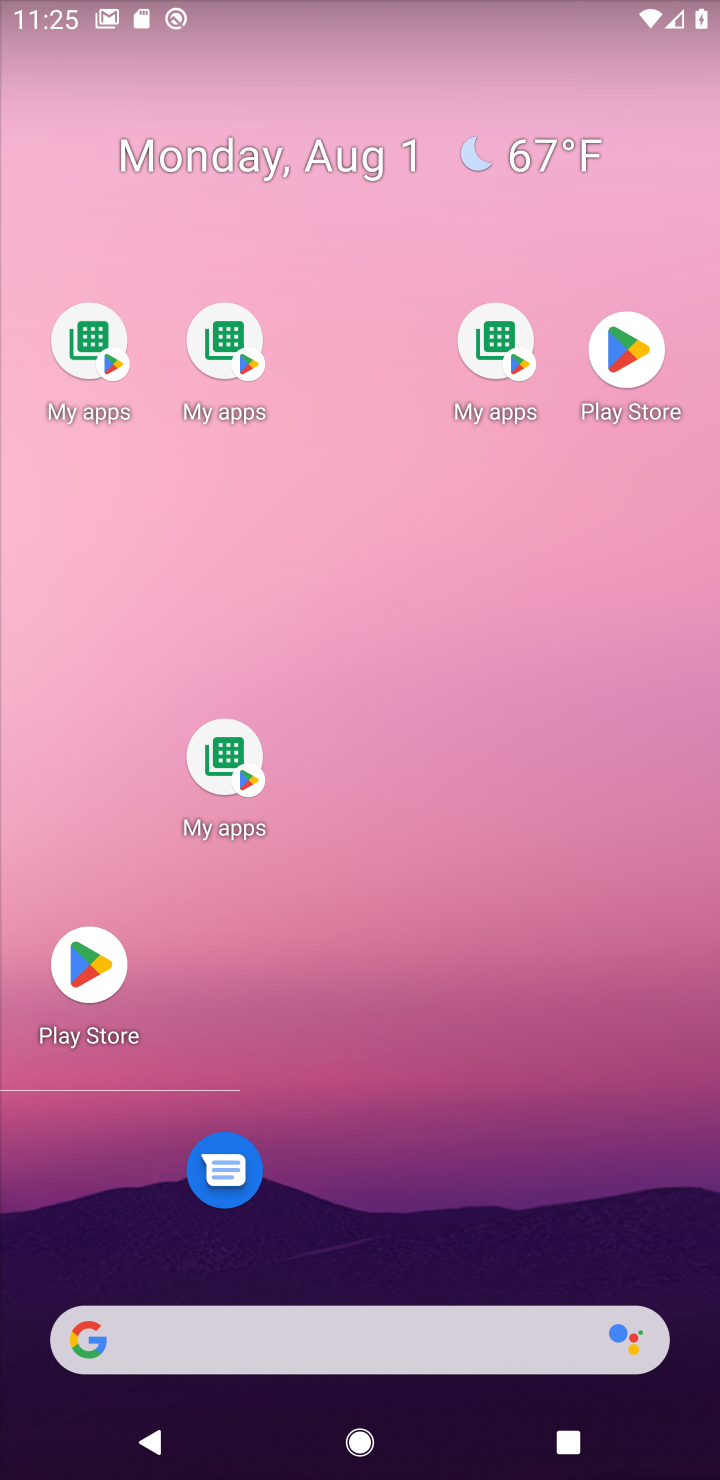
Step 34: drag from (657, 359) to (128, 327)
Your task to perform on an android device: open app "The Home Depot" (install if not already installed) Image 35: 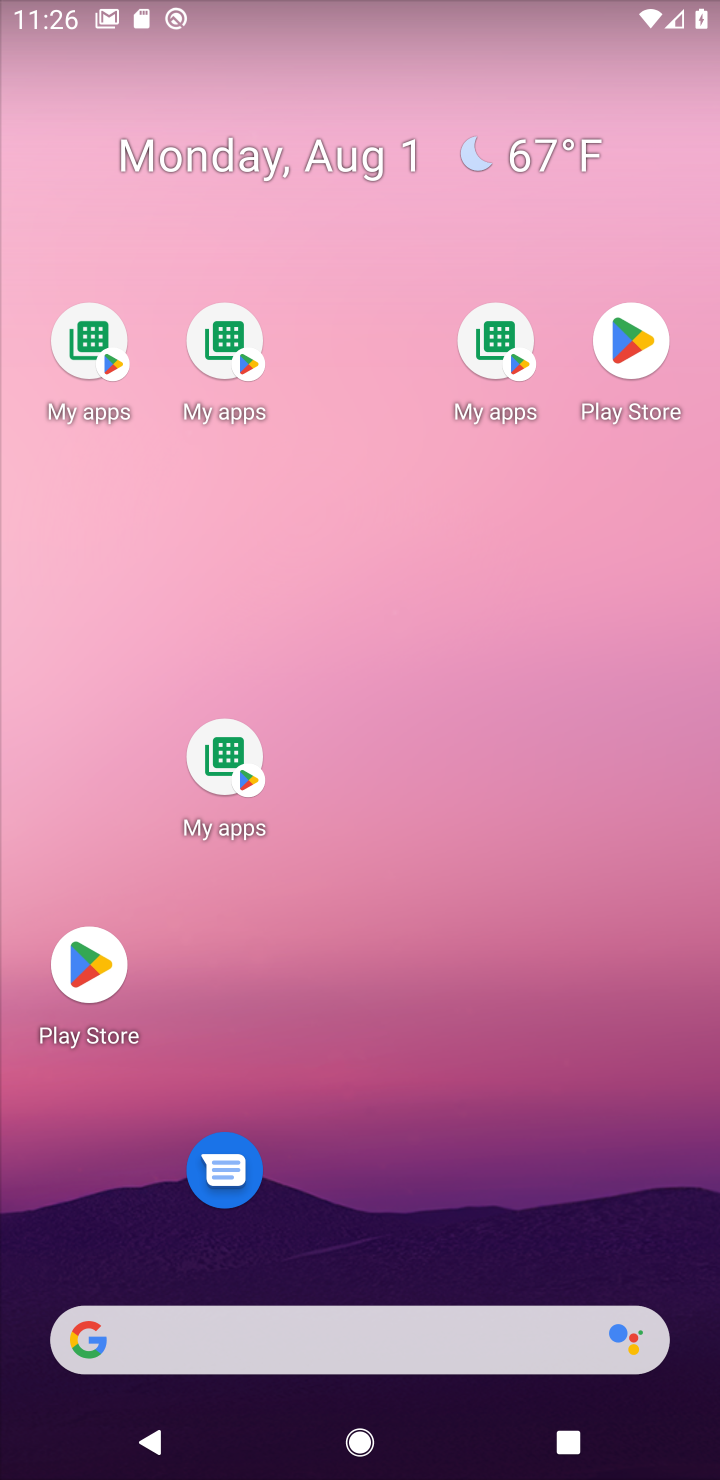
Step 35: drag from (333, 57) to (535, 523)
Your task to perform on an android device: open app "The Home Depot" (install if not already installed) Image 36: 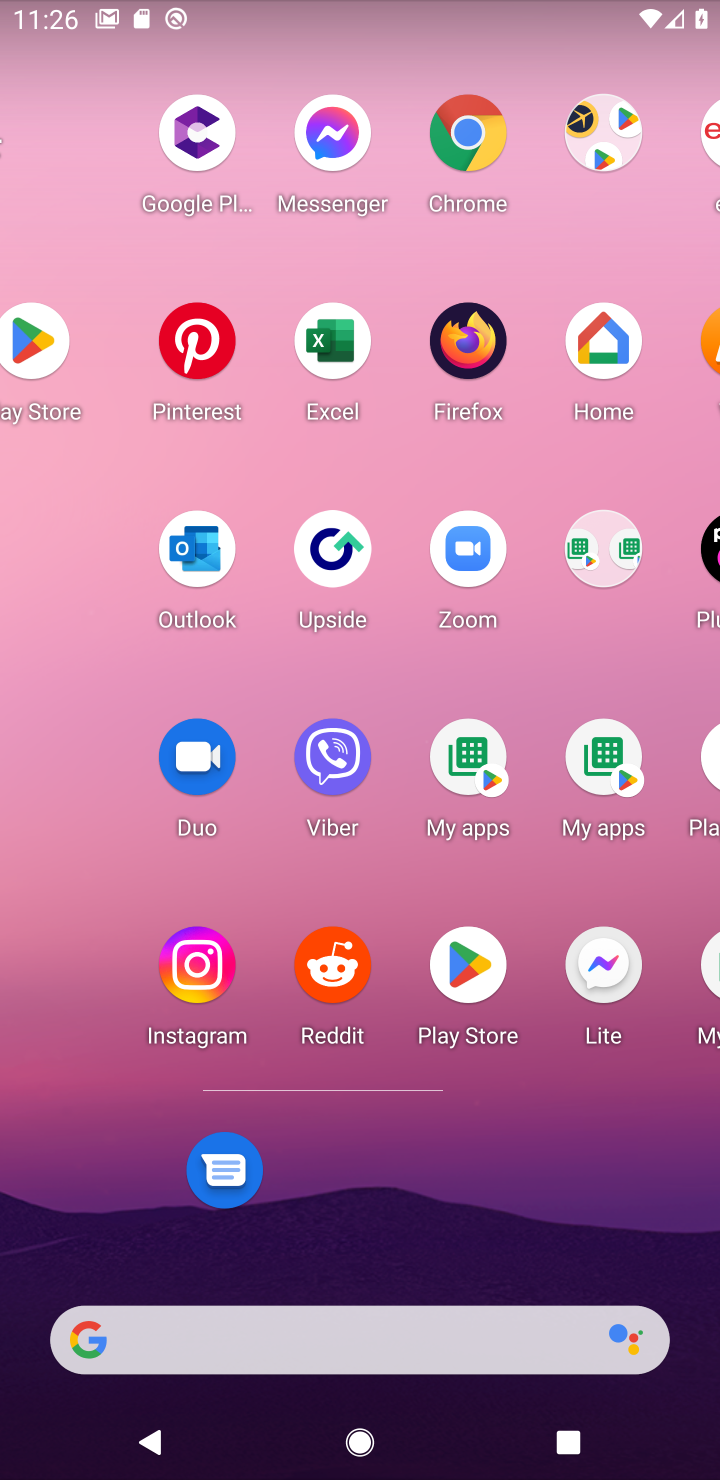
Step 36: click (614, 376)
Your task to perform on an android device: open app "The Home Depot" (install if not already installed) Image 37: 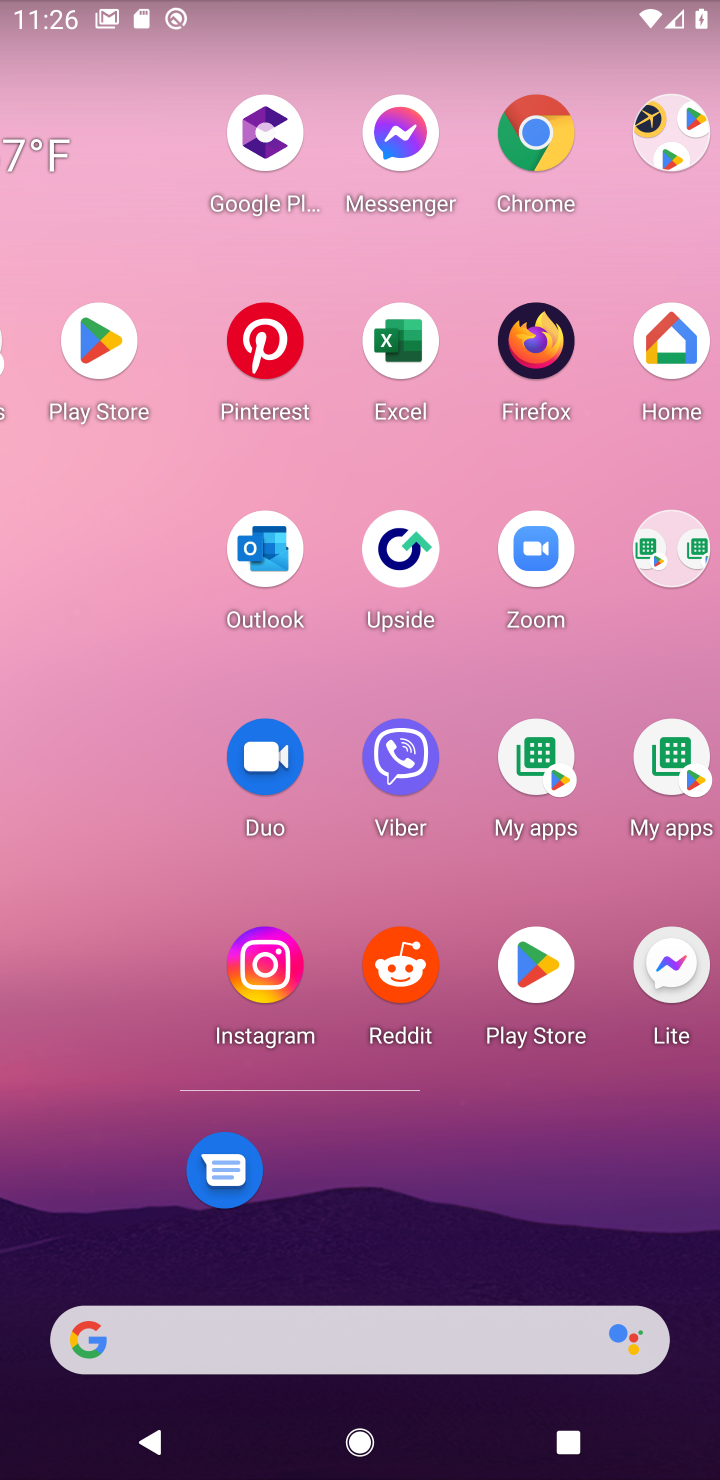
Step 37: click (625, 331)
Your task to perform on an android device: open app "The Home Depot" (install if not already installed) Image 38: 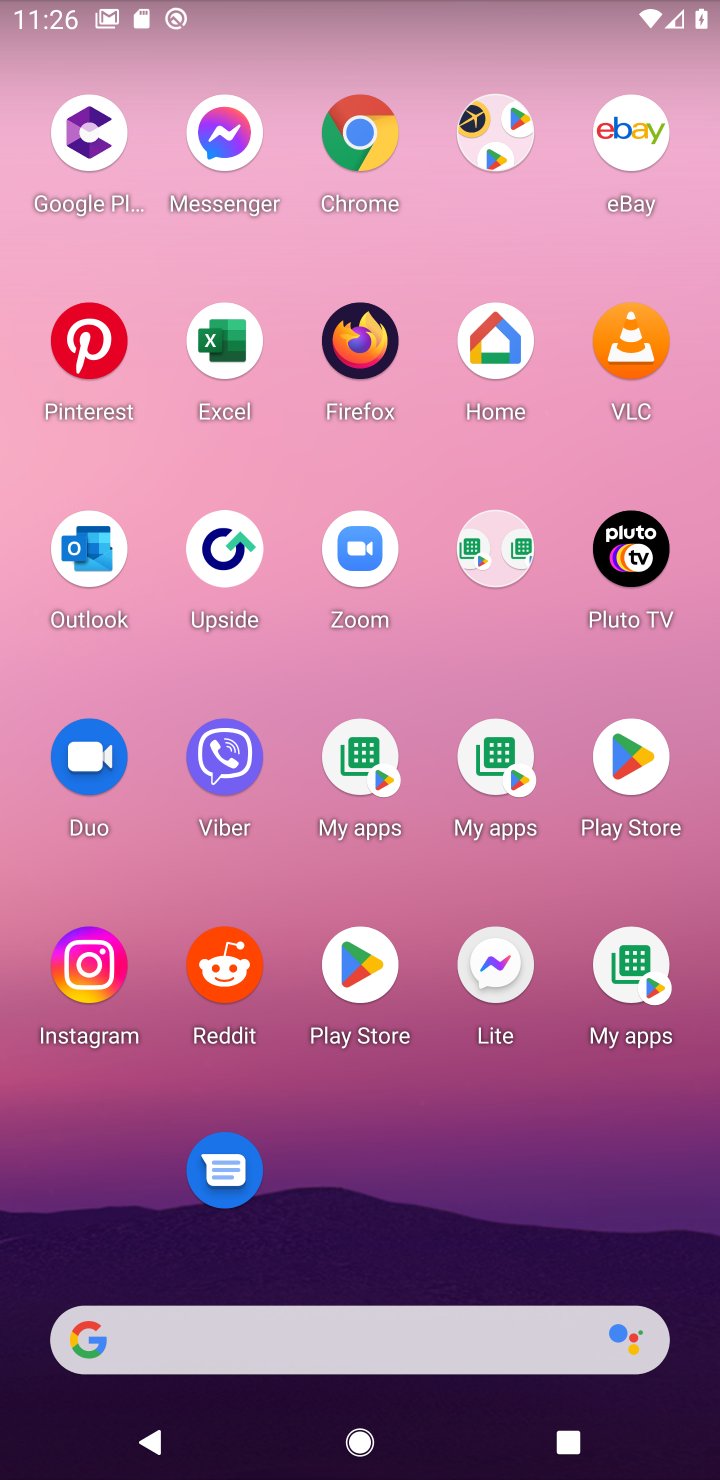
Step 38: drag from (619, 754) to (687, 808)
Your task to perform on an android device: open app "The Home Depot" (install if not already installed) Image 39: 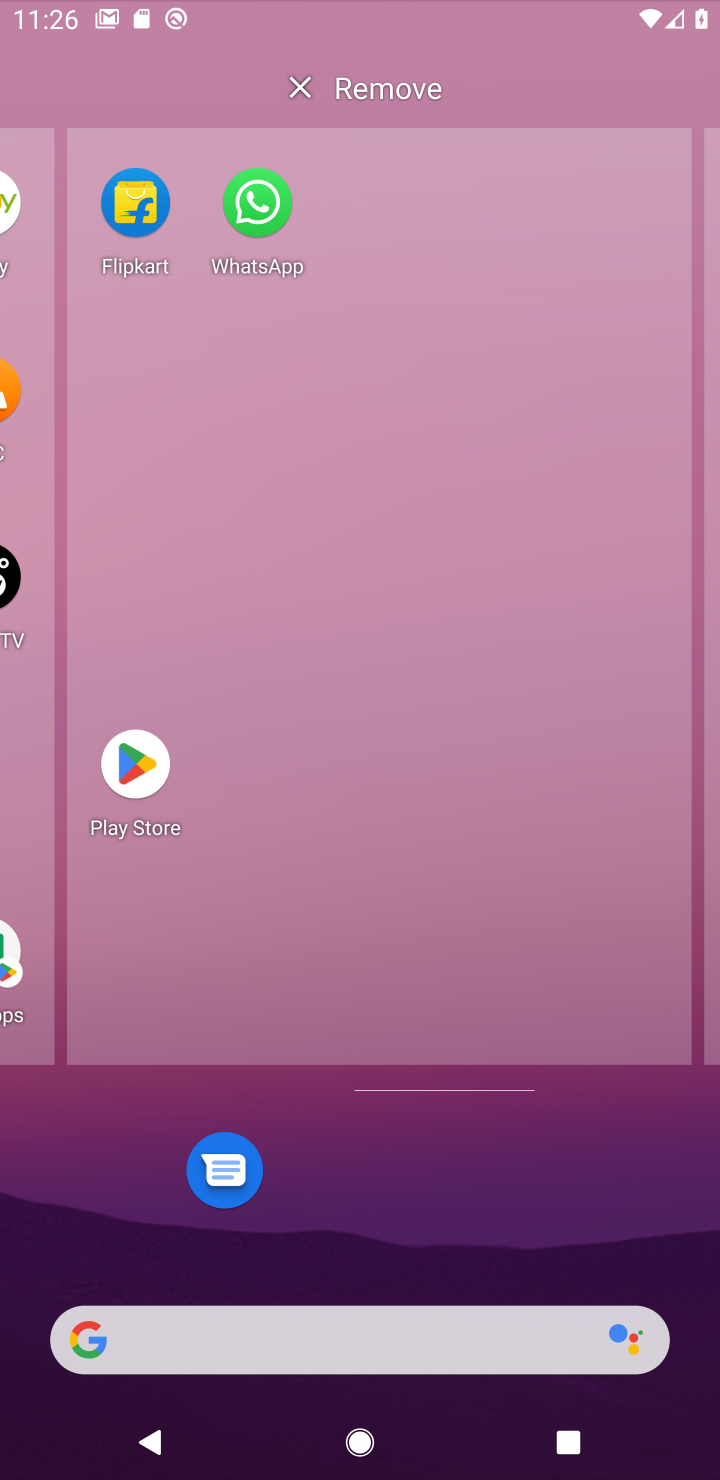
Step 39: click (631, 751)
Your task to perform on an android device: open app "The Home Depot" (install if not already installed) Image 40: 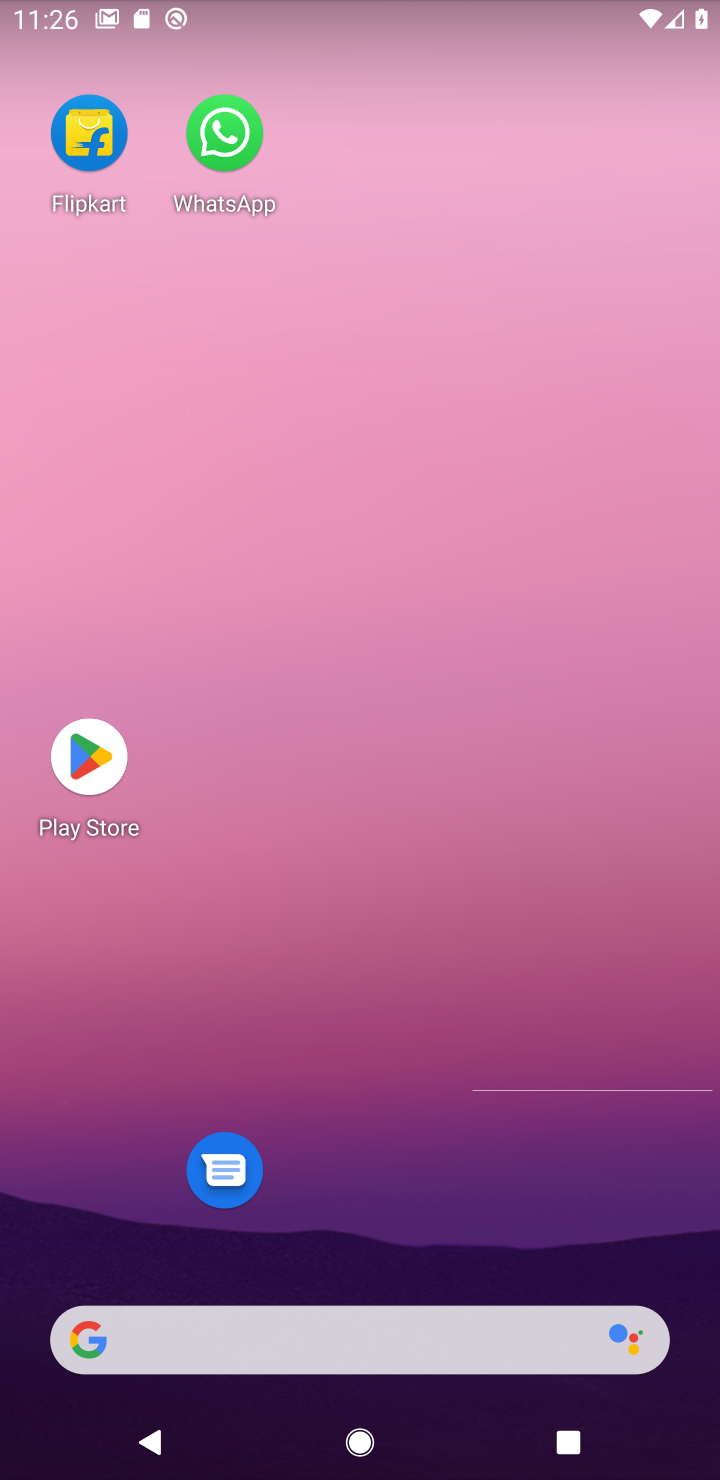
Step 40: drag from (293, 858) to (113, 307)
Your task to perform on an android device: open app "The Home Depot" (install if not already installed) Image 41: 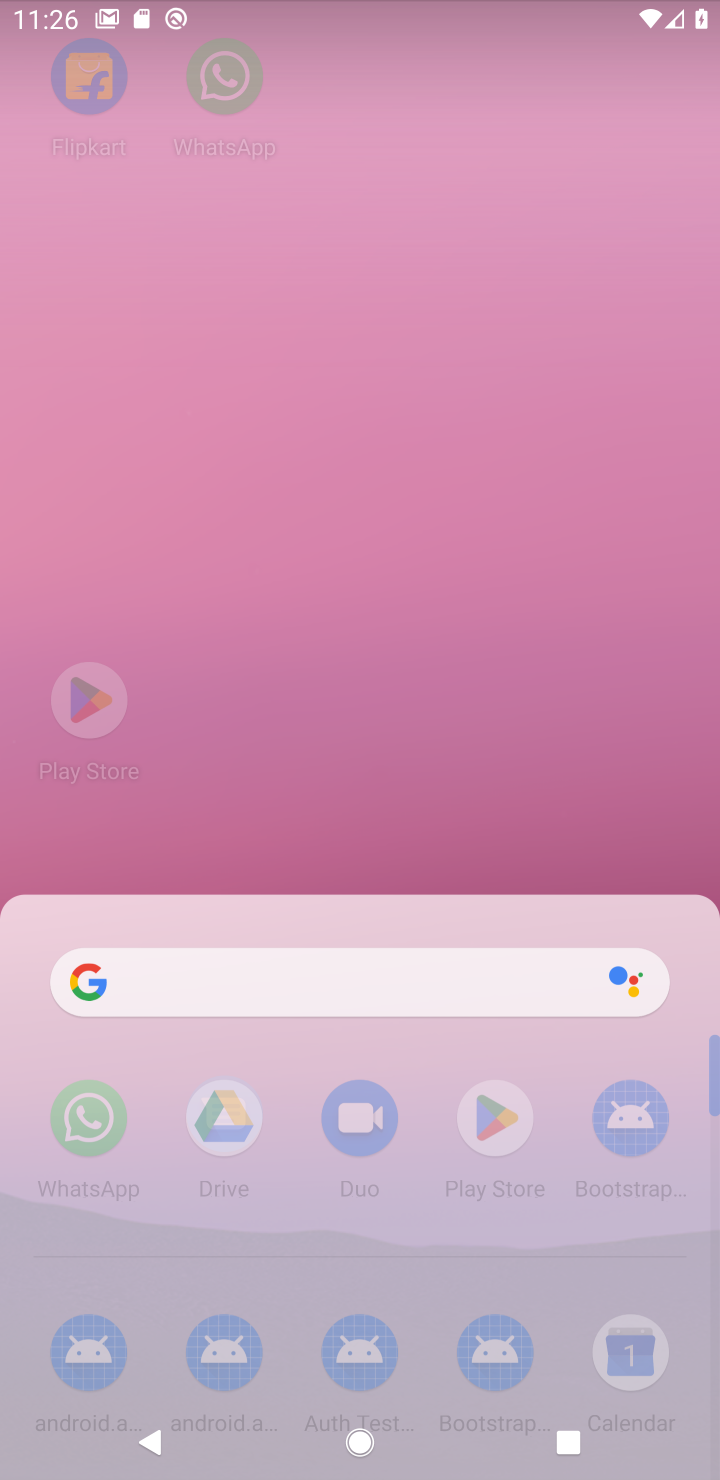
Step 41: drag from (204, 989) to (154, 383)
Your task to perform on an android device: open app "The Home Depot" (install if not already installed) Image 42: 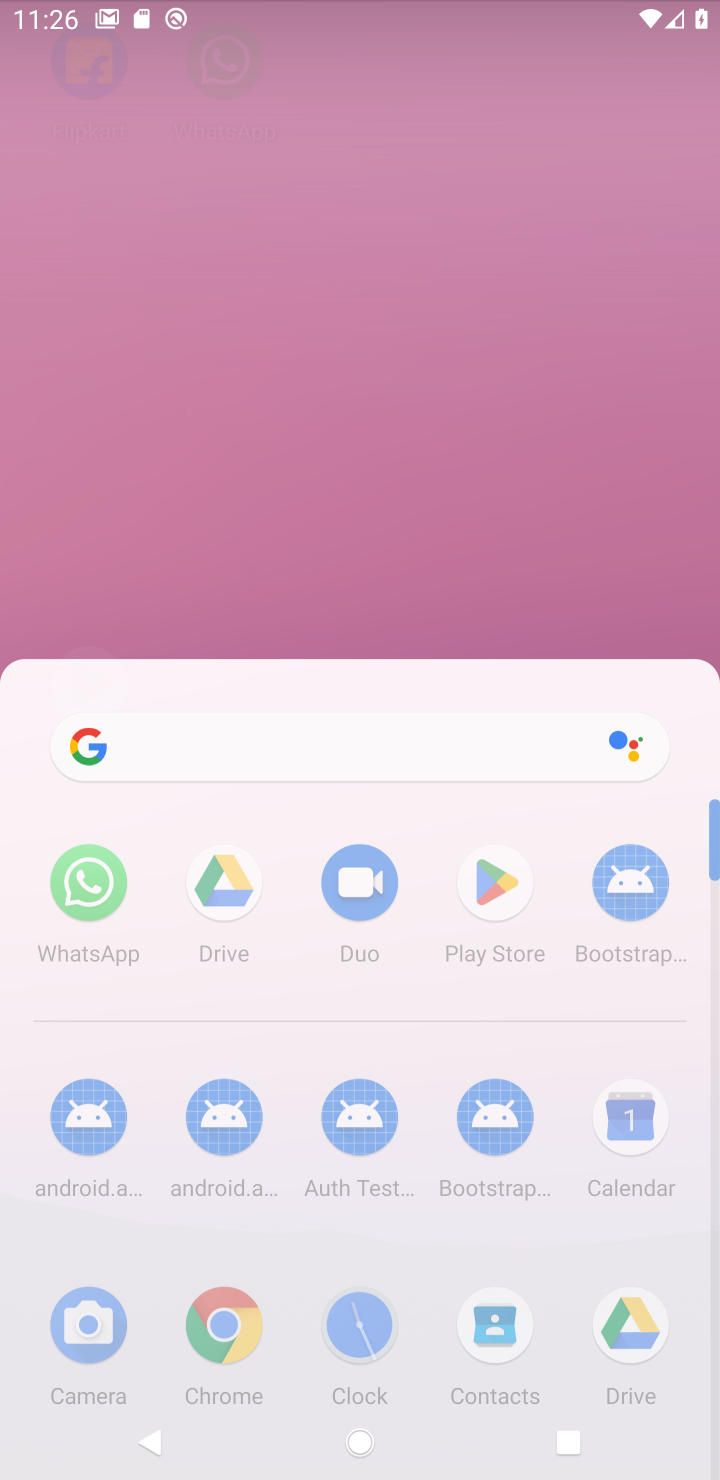
Step 42: drag from (154, 286) to (329, 161)
Your task to perform on an android device: open app "The Home Depot" (install if not already installed) Image 43: 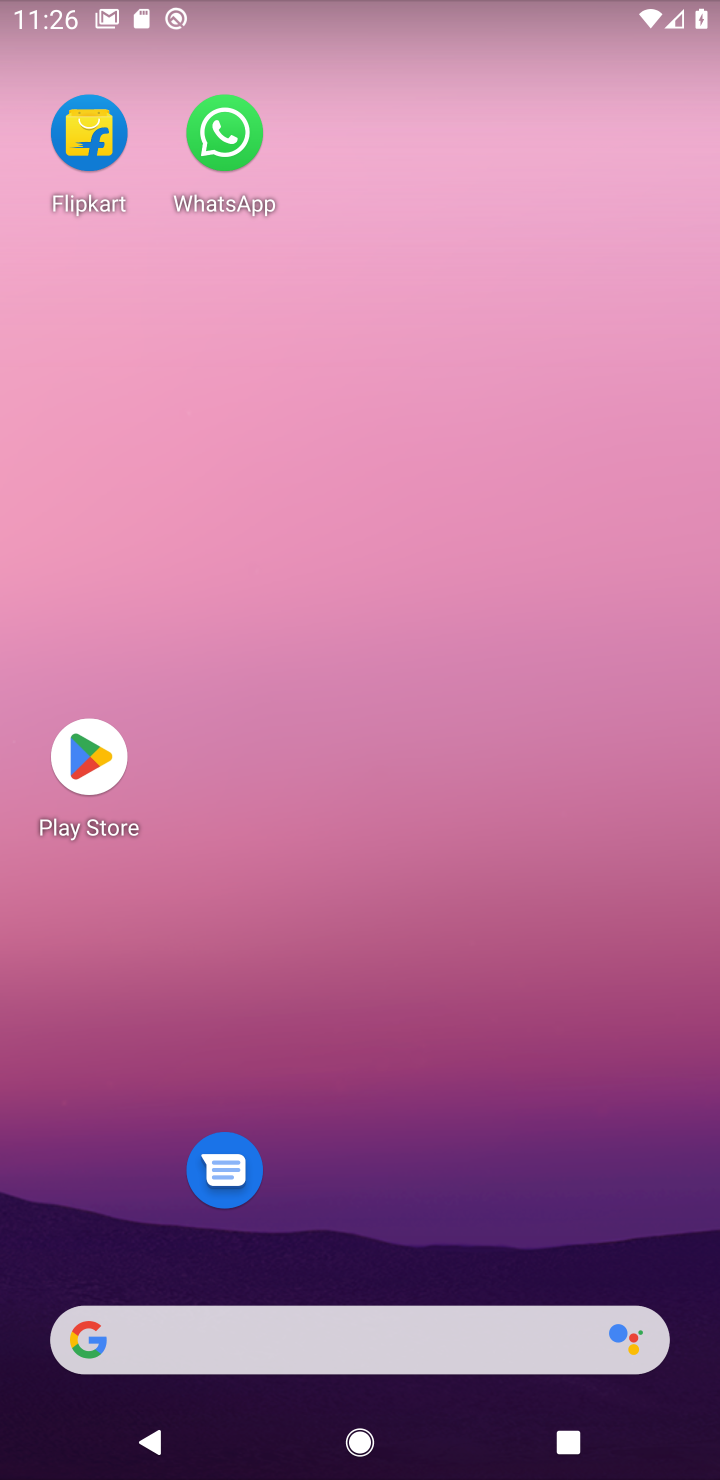
Step 43: drag from (367, 743) to (70, 11)
Your task to perform on an android device: open app "The Home Depot" (install if not already installed) Image 44: 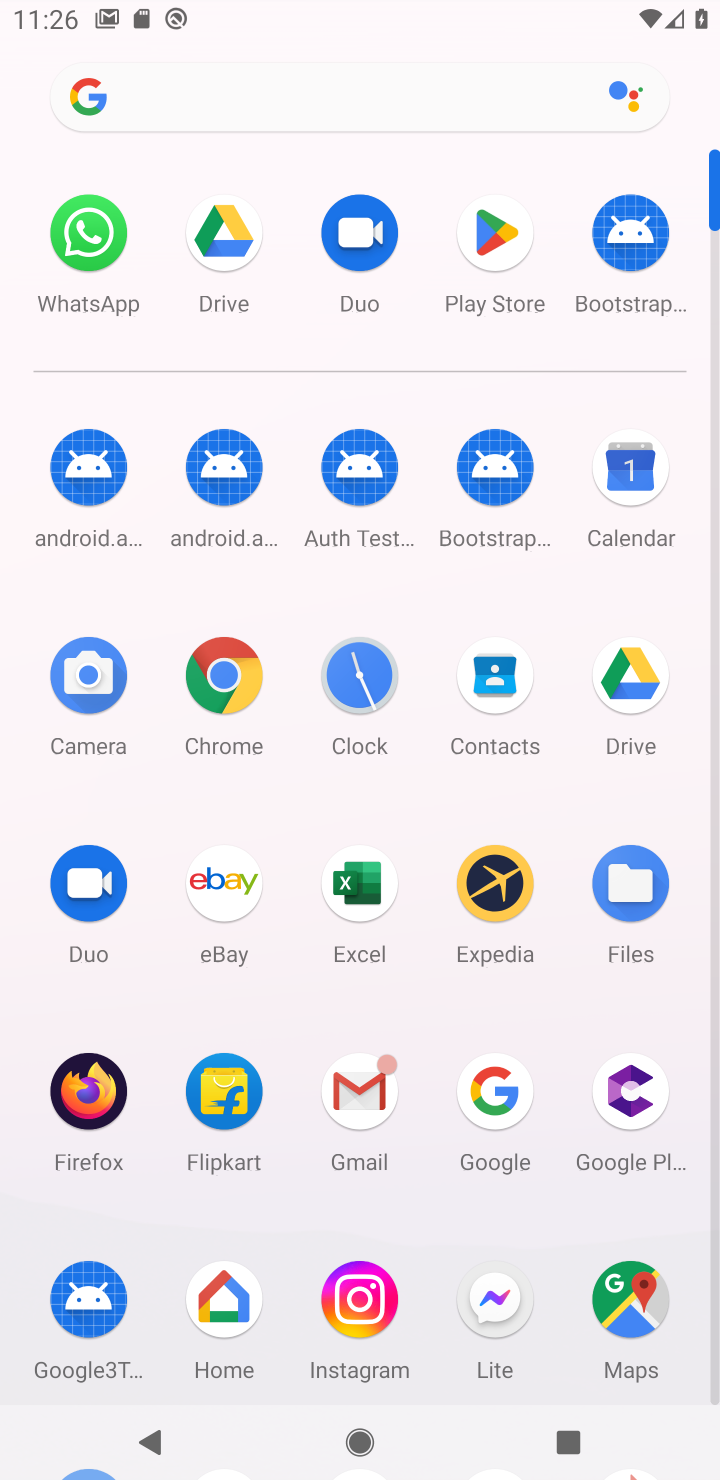
Step 44: drag from (332, 1101) to (477, 55)
Your task to perform on an android device: open app "The Home Depot" (install if not already installed) Image 45: 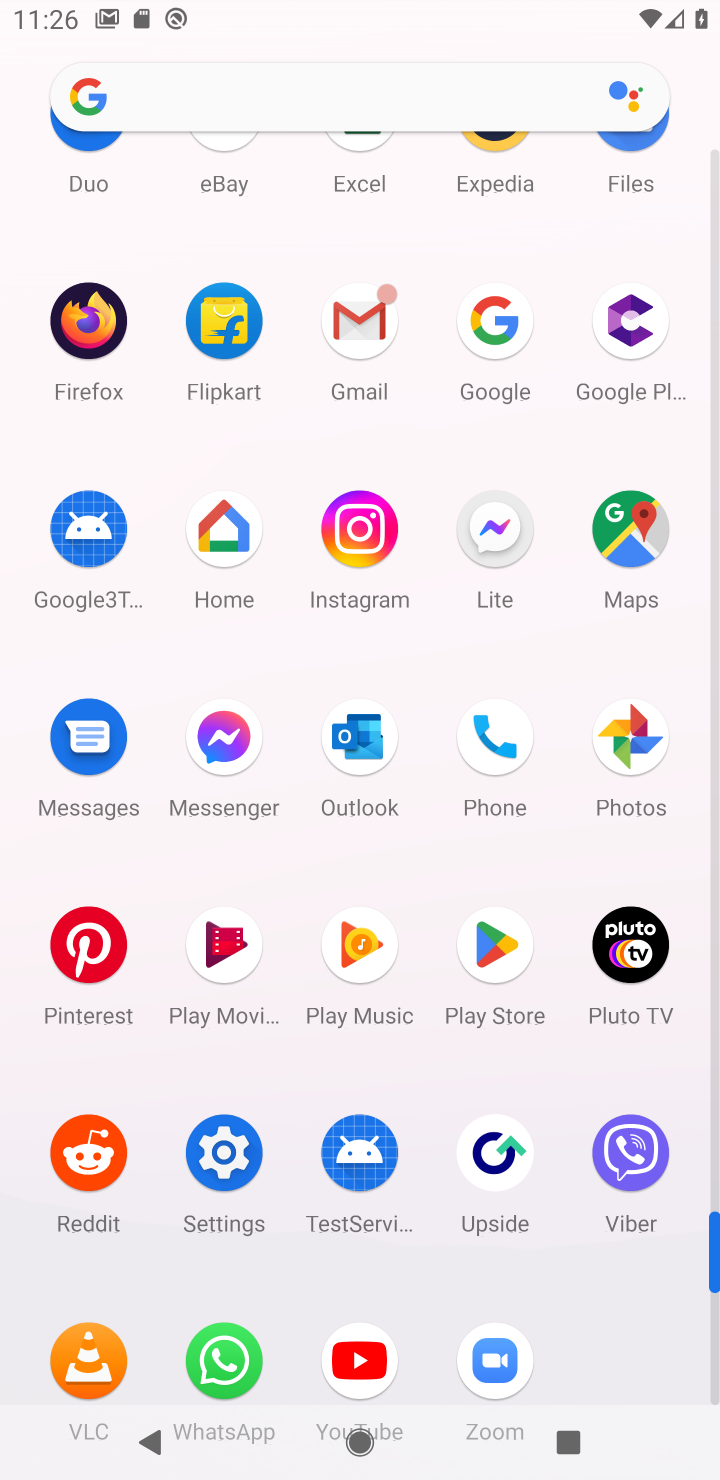
Step 45: drag from (288, 1065) to (190, 395)
Your task to perform on an android device: open app "The Home Depot" (install if not already installed) Image 46: 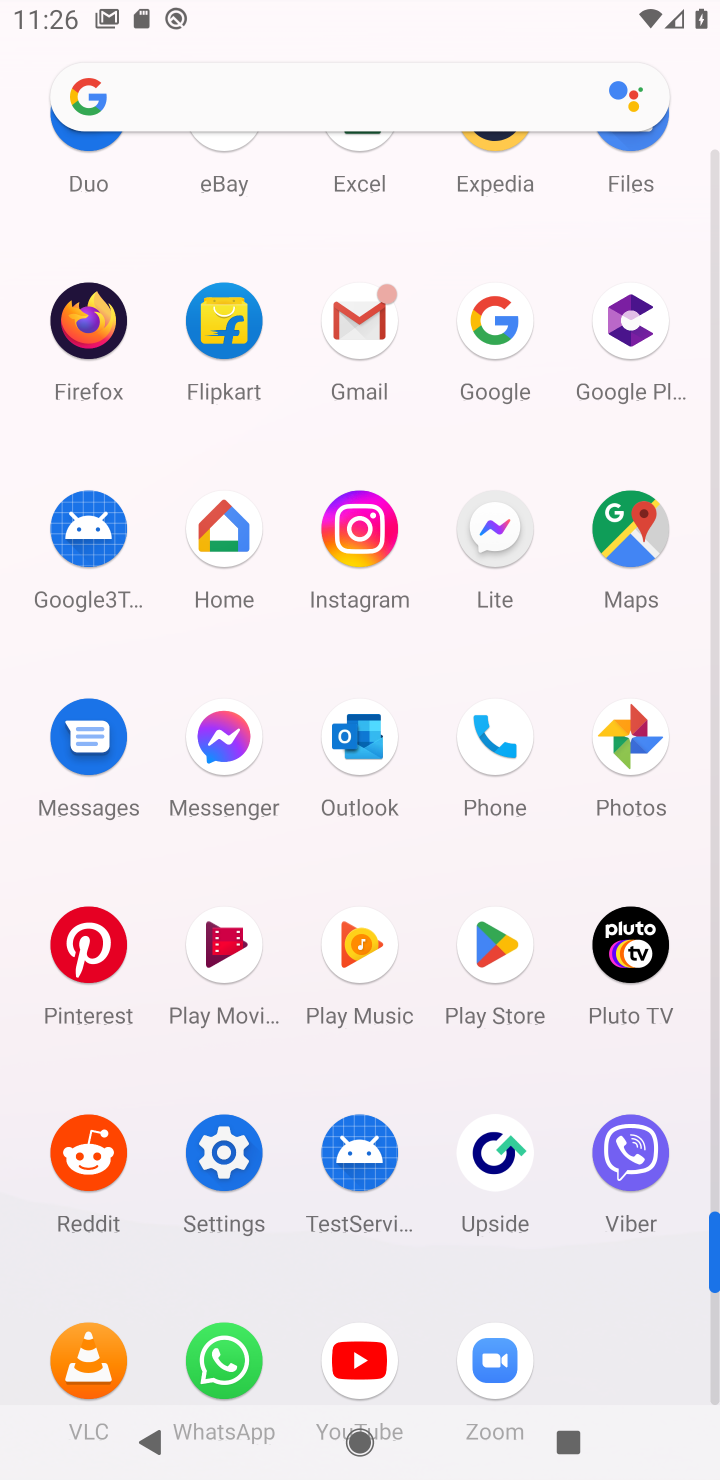
Step 46: drag from (447, 542) to (453, 1020)
Your task to perform on an android device: open app "The Home Depot" (install if not already installed) Image 47: 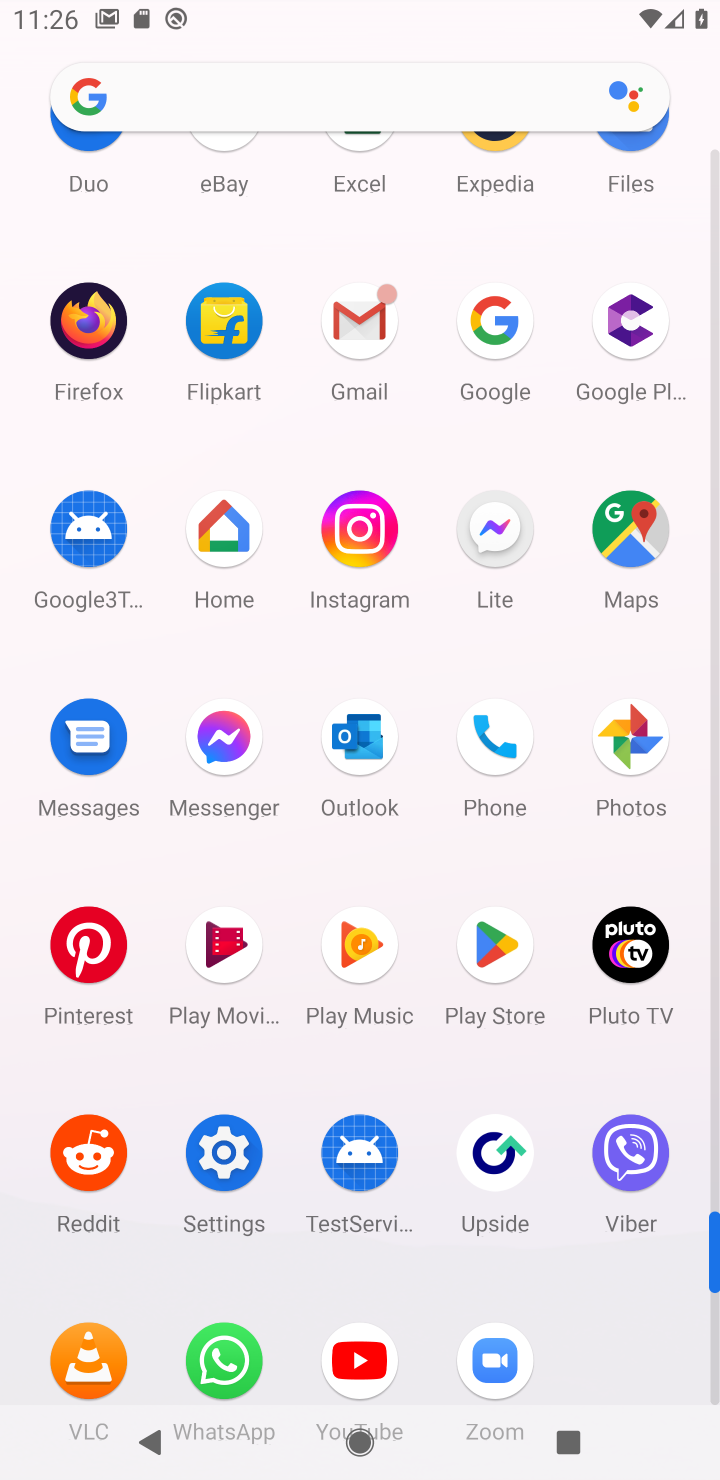
Step 47: drag from (439, 1105) to (454, 1232)
Your task to perform on an android device: open app "The Home Depot" (install if not already installed) Image 48: 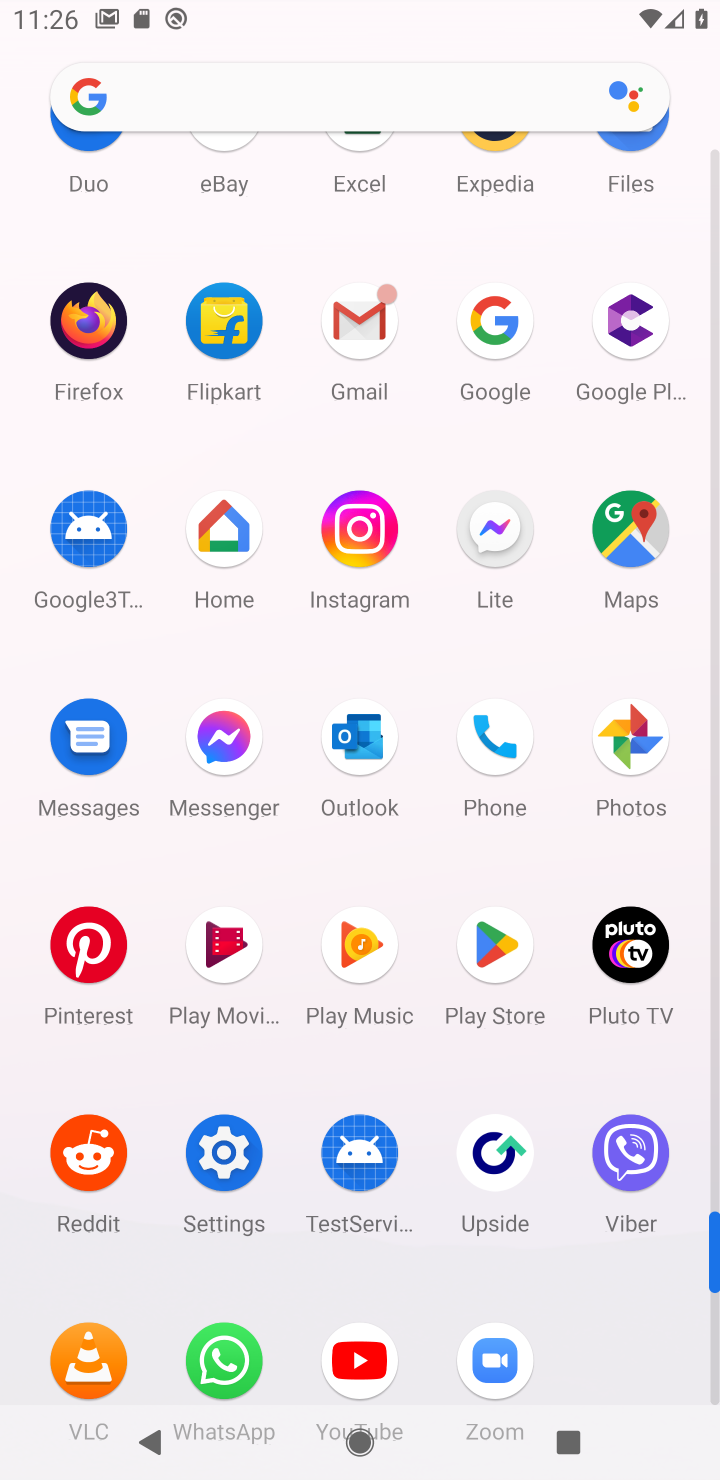
Step 48: drag from (395, 437) to (435, 1336)
Your task to perform on an android device: open app "The Home Depot" (install if not already installed) Image 49: 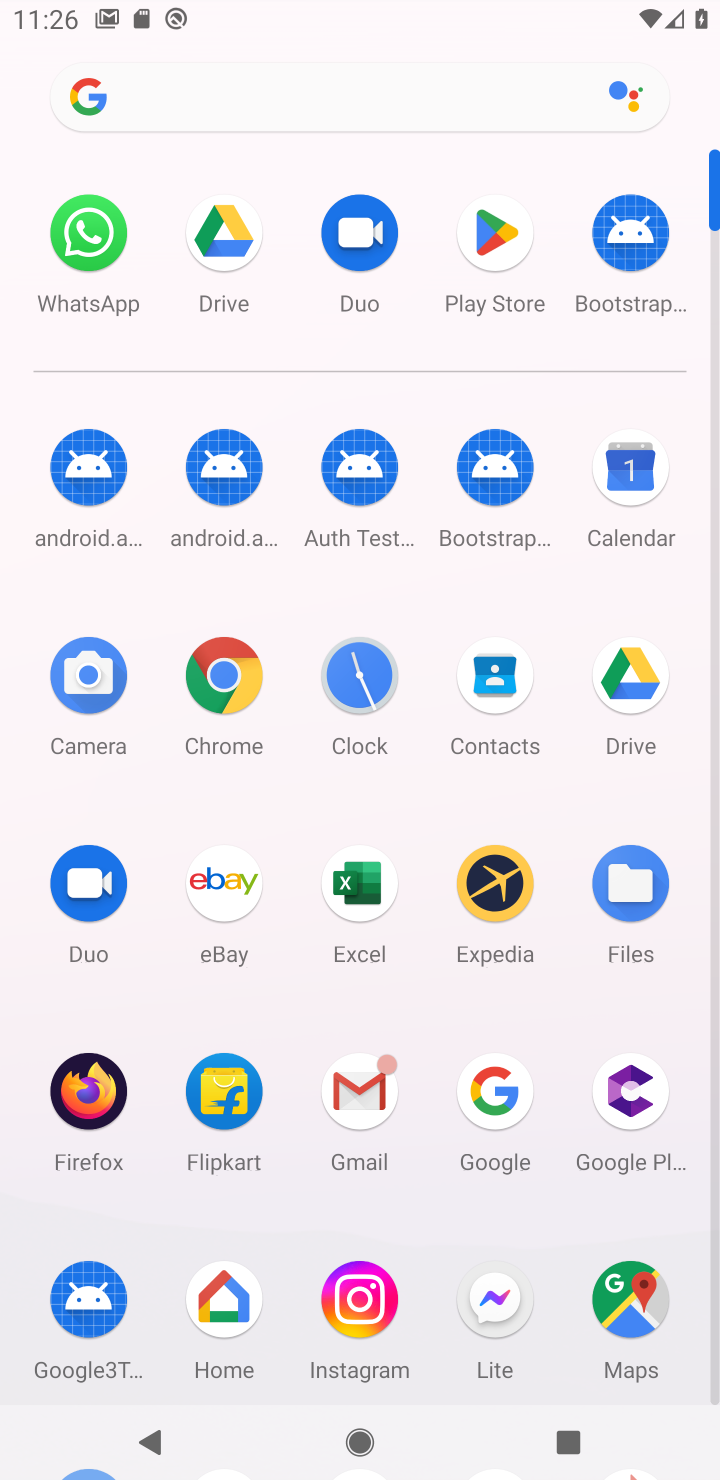
Step 49: click (490, 235)
Your task to perform on an android device: open app "The Home Depot" (install if not already installed) Image 50: 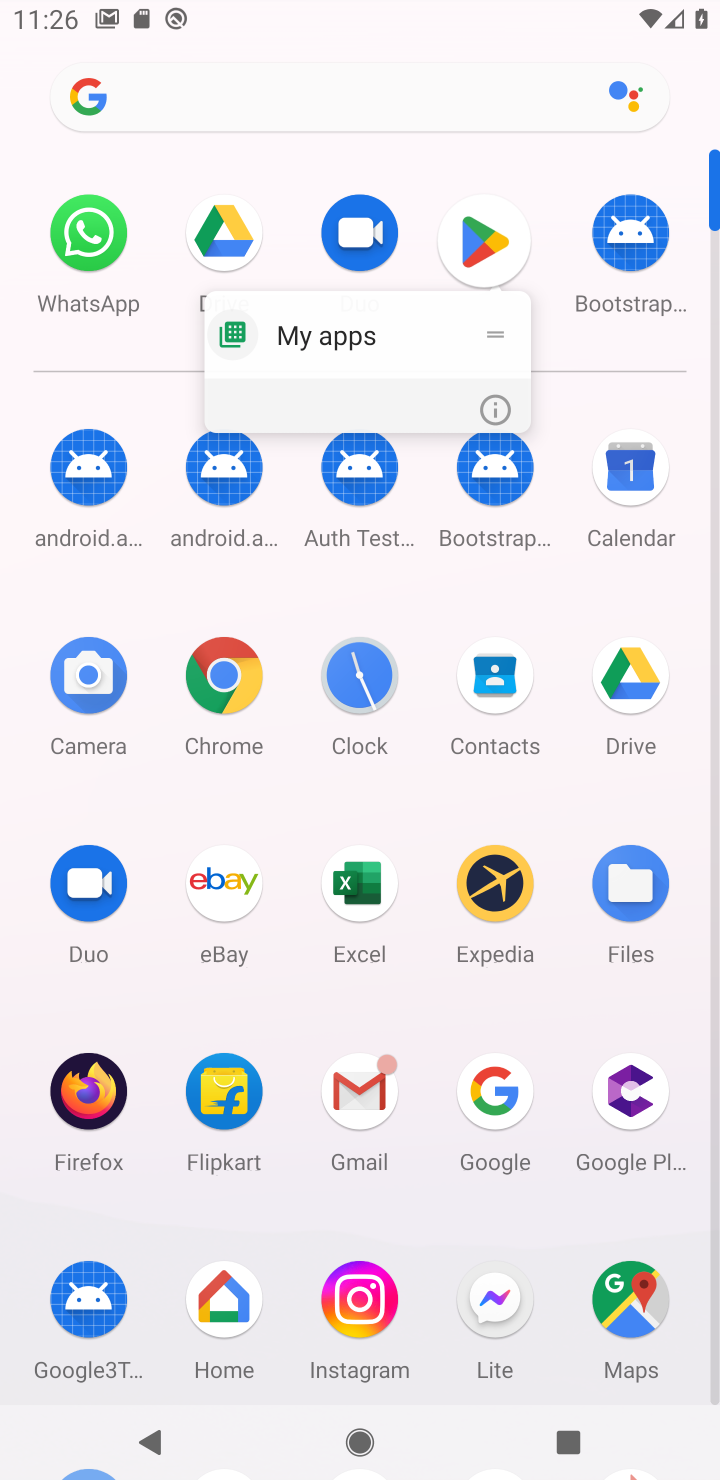
Step 50: click (332, 344)
Your task to perform on an android device: open app "The Home Depot" (install if not already installed) Image 51: 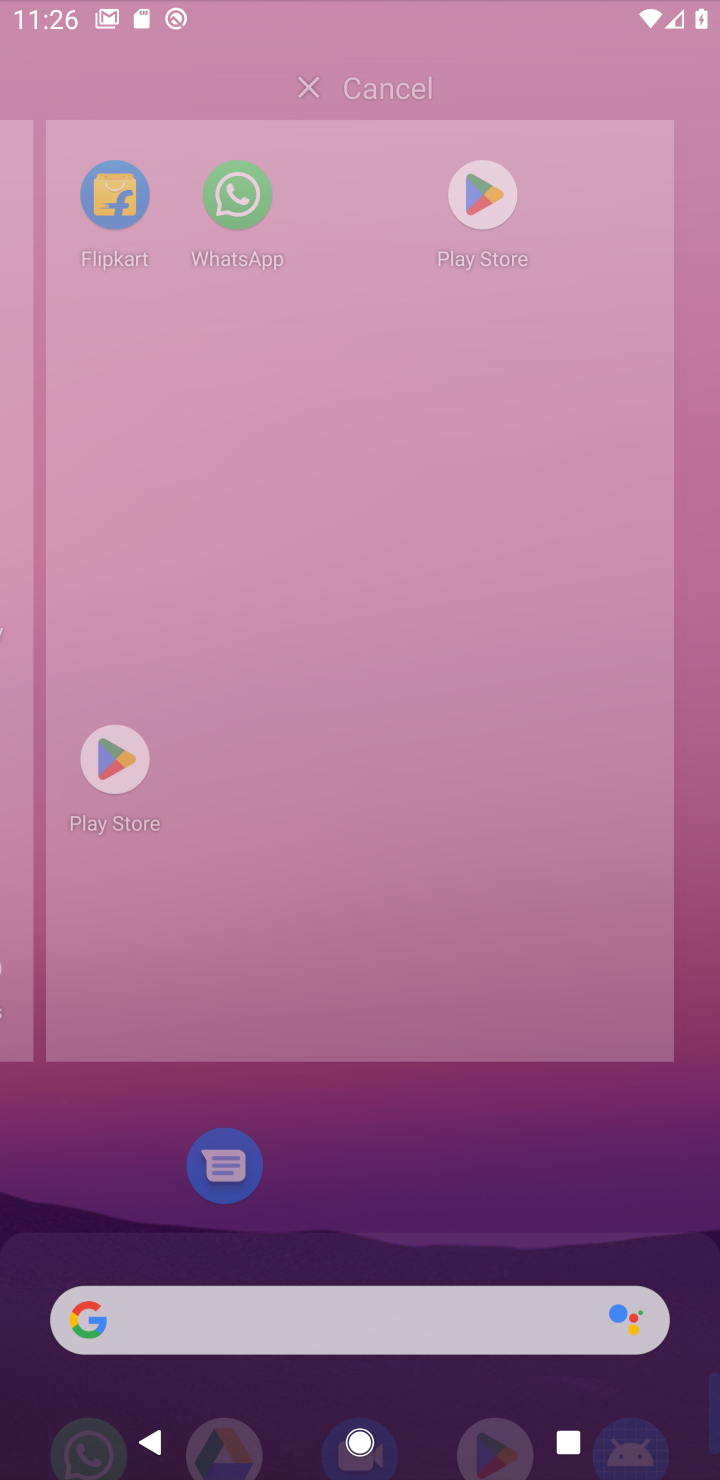
Step 51: click (342, 332)
Your task to perform on an android device: open app "The Home Depot" (install if not already installed) Image 52: 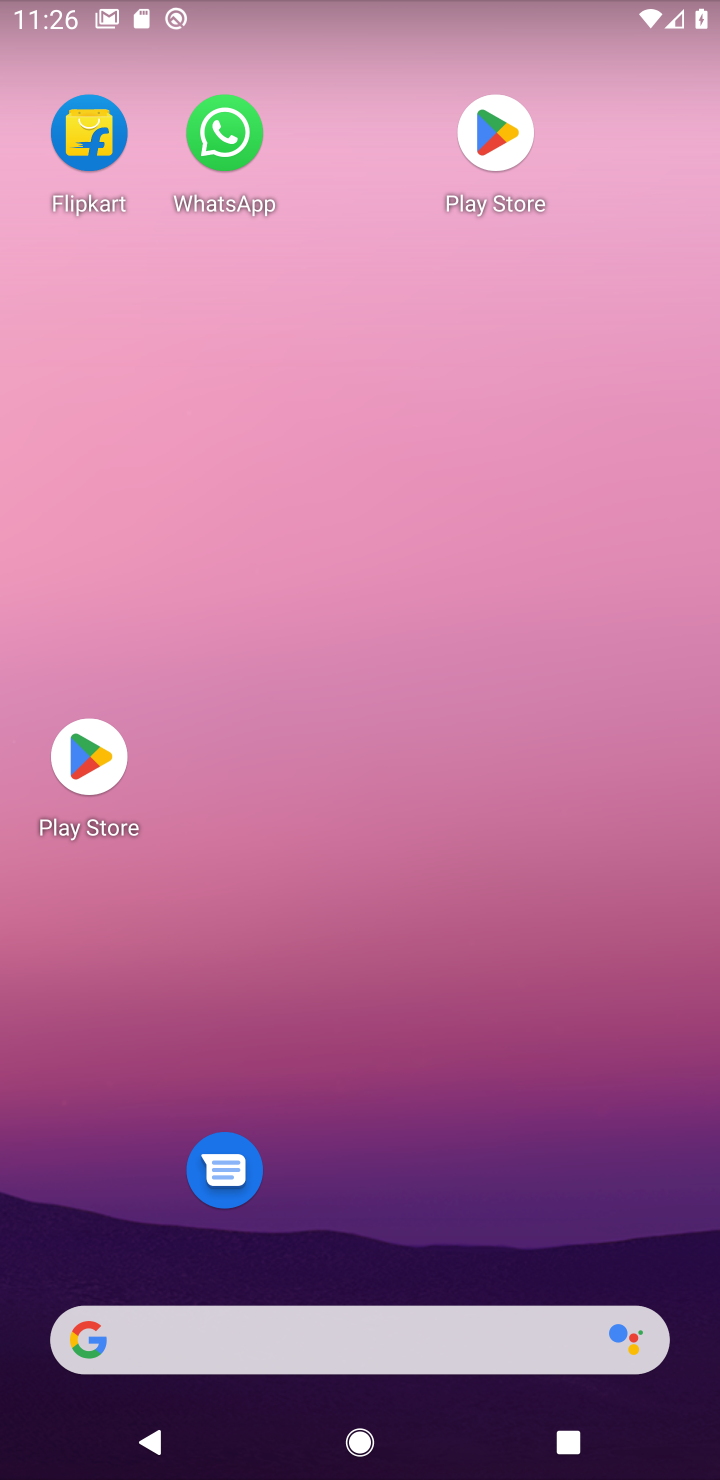
Step 52: click (475, 138)
Your task to perform on an android device: open app "The Home Depot" (install if not already installed) Image 53: 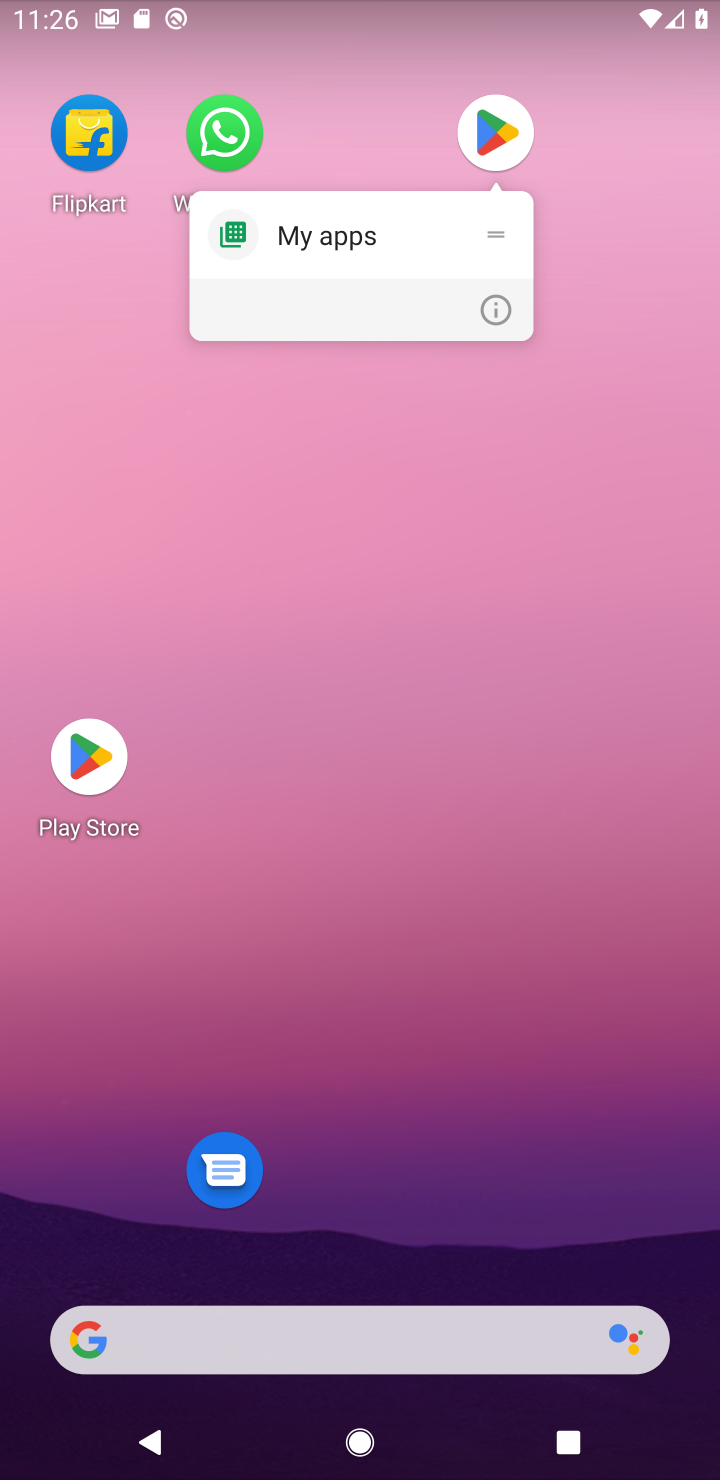
Step 53: click (297, 223)
Your task to perform on an android device: open app "The Home Depot" (install if not already installed) Image 54: 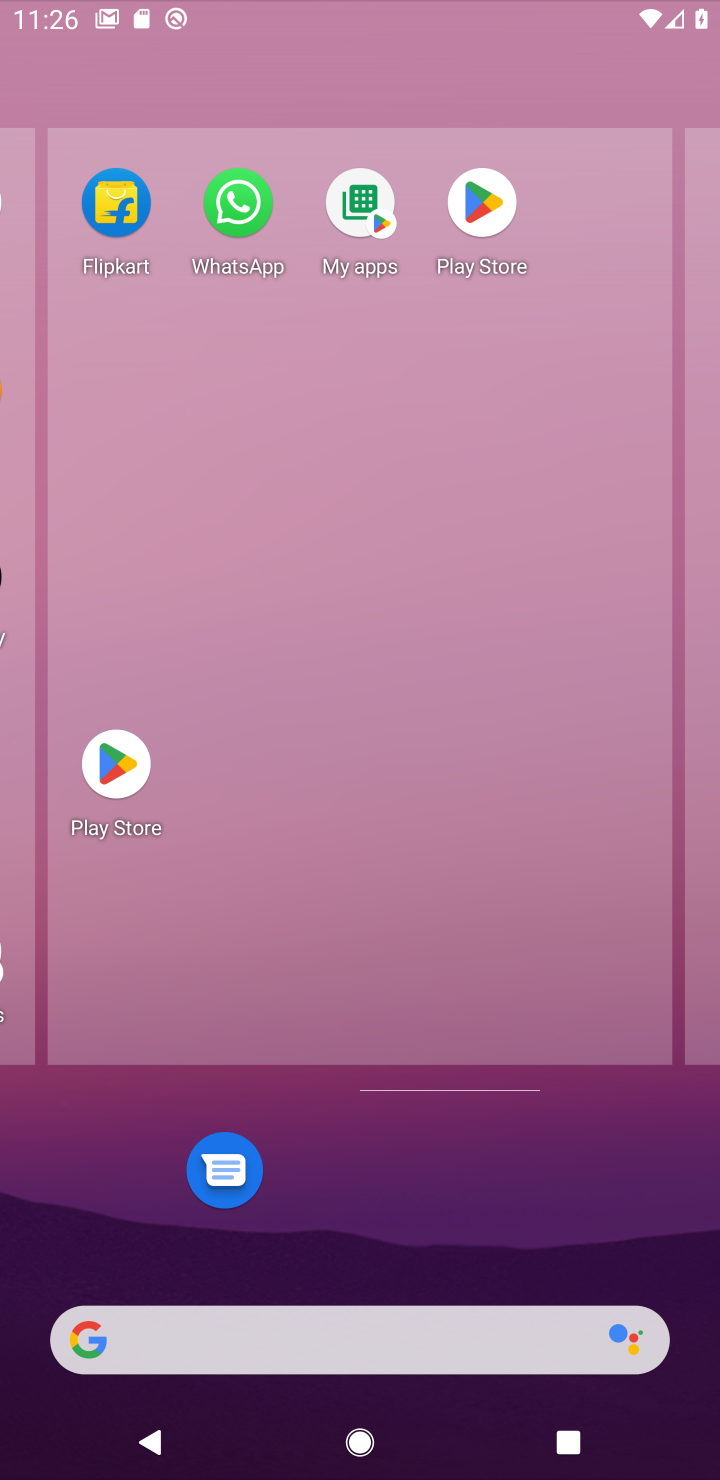
Step 54: click (493, 196)
Your task to perform on an android device: open app "The Home Depot" (install if not already installed) Image 55: 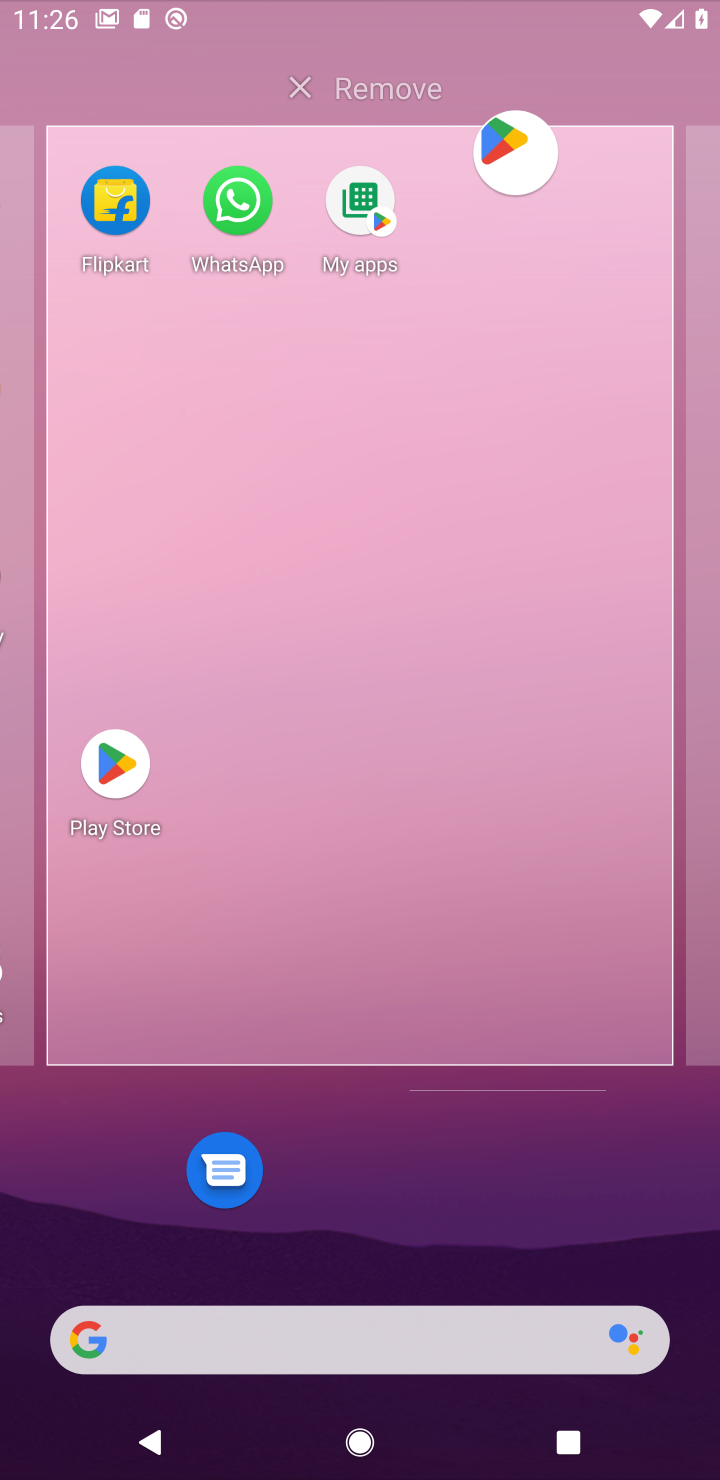
Step 55: click (502, 153)
Your task to perform on an android device: open app "The Home Depot" (install if not already installed) Image 56: 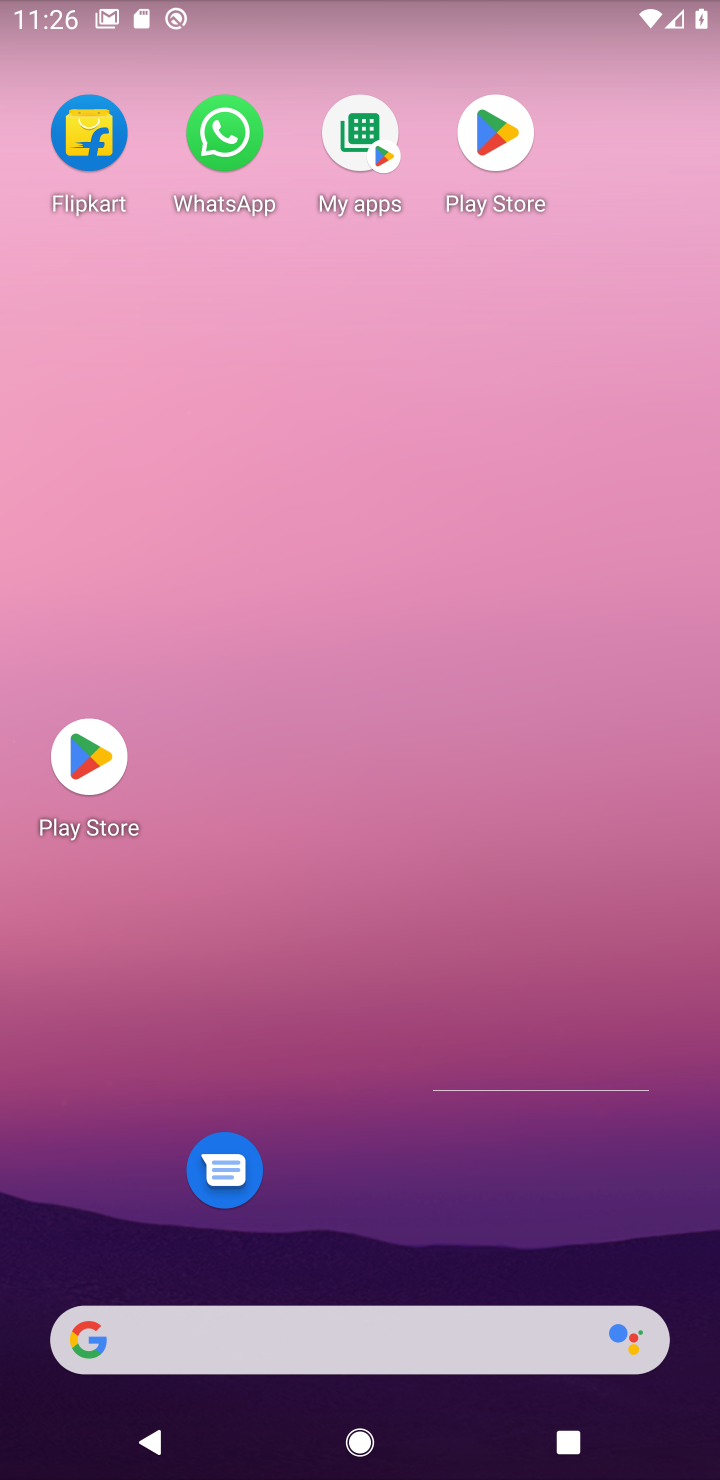
Step 56: click (513, 151)
Your task to perform on an android device: open app "The Home Depot" (install if not already installed) Image 57: 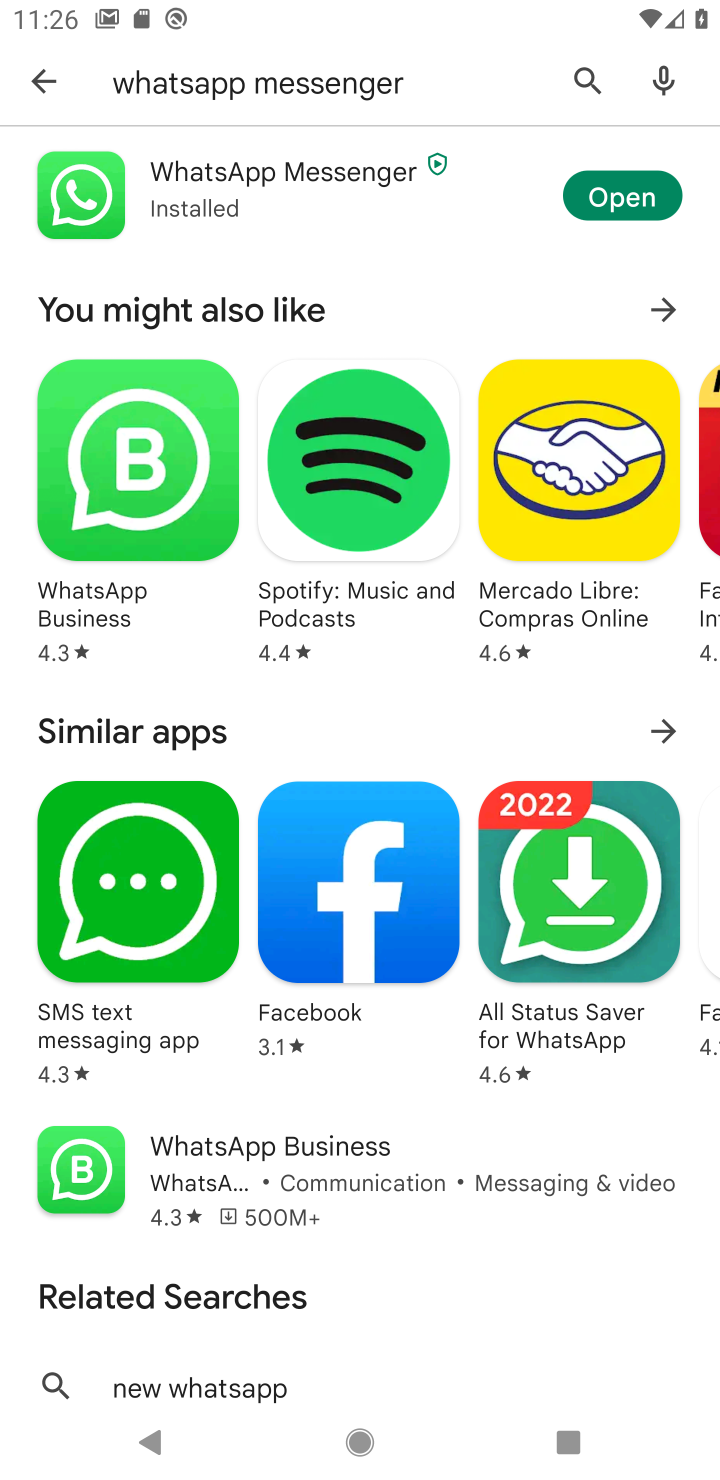
Step 57: click (587, 114)
Your task to perform on an android device: open app "The Home Depot" (install if not already installed) Image 58: 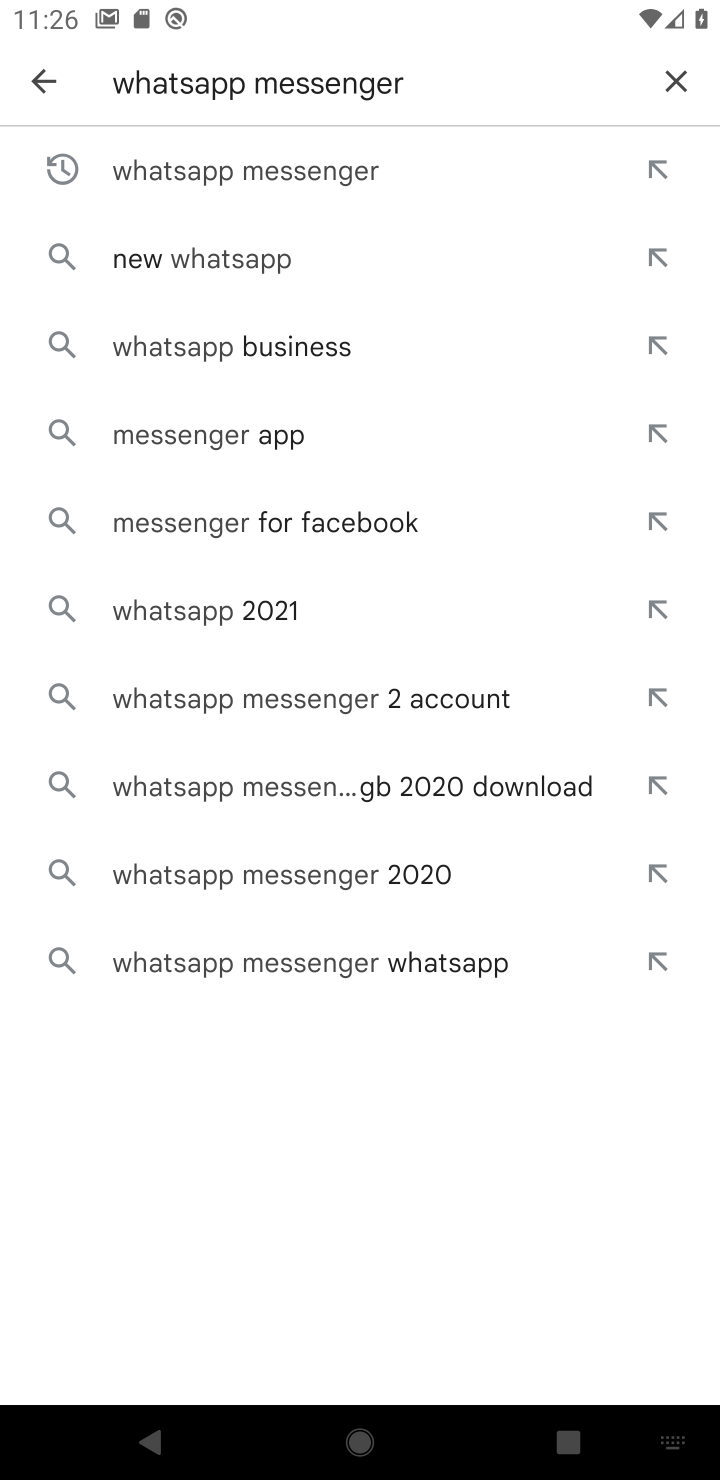
Step 58: click (674, 64)
Your task to perform on an android device: open app "The Home Depot" (install if not already installed) Image 59: 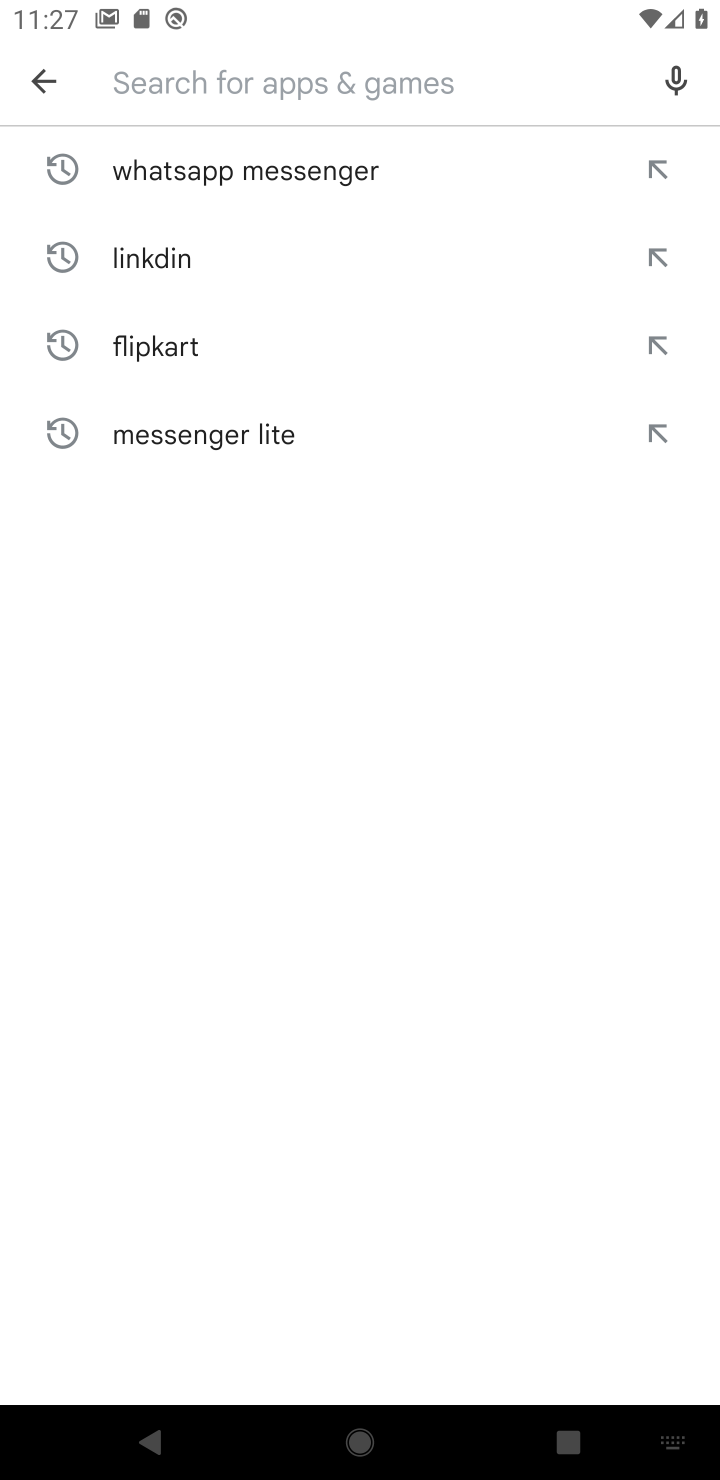
Step 59: type "The Home Depot"
Your task to perform on an android device: open app "The Home Depot" (install if not already installed) Image 60: 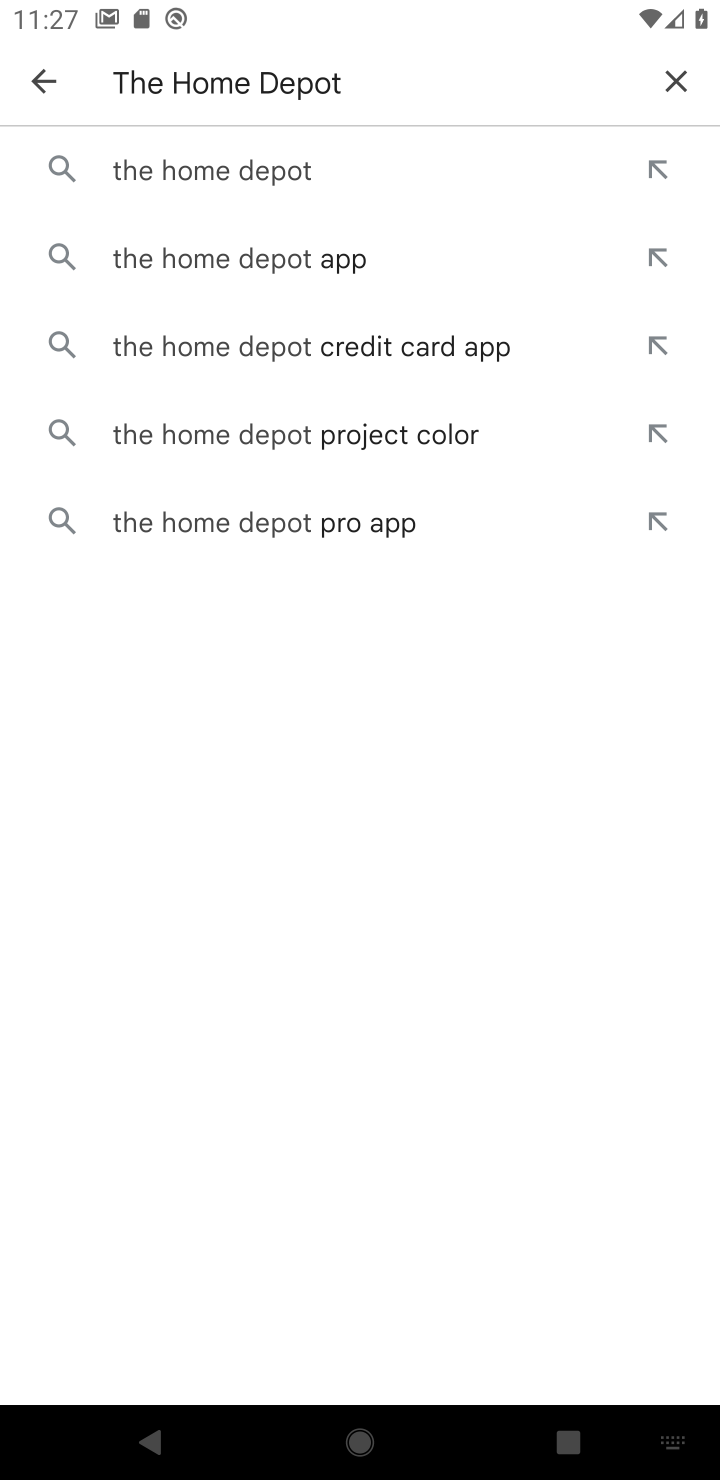
Step 60: click (251, 160)
Your task to perform on an android device: open app "The Home Depot" (install if not already installed) Image 61: 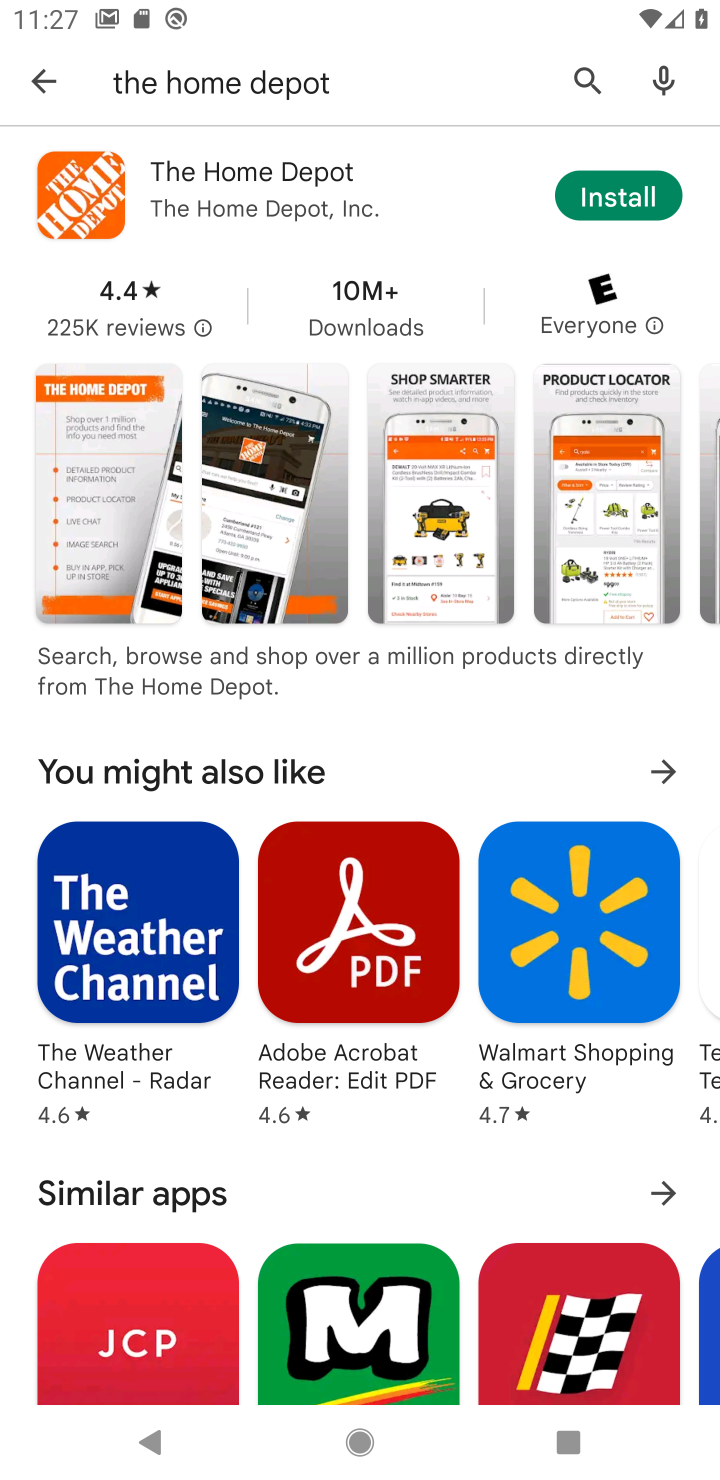
Step 61: click (621, 172)
Your task to perform on an android device: open app "The Home Depot" (install if not already installed) Image 62: 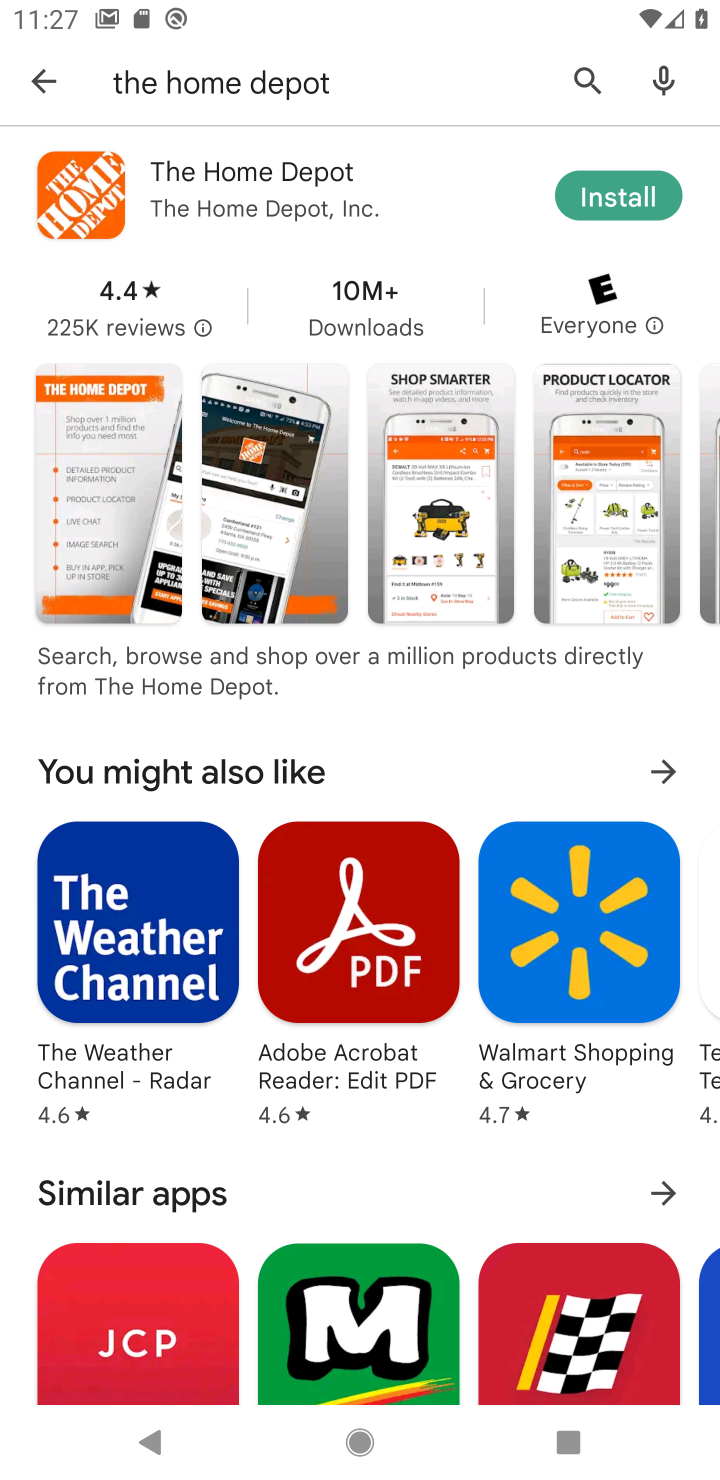
Step 62: click (618, 181)
Your task to perform on an android device: open app "The Home Depot" (install if not already installed) Image 63: 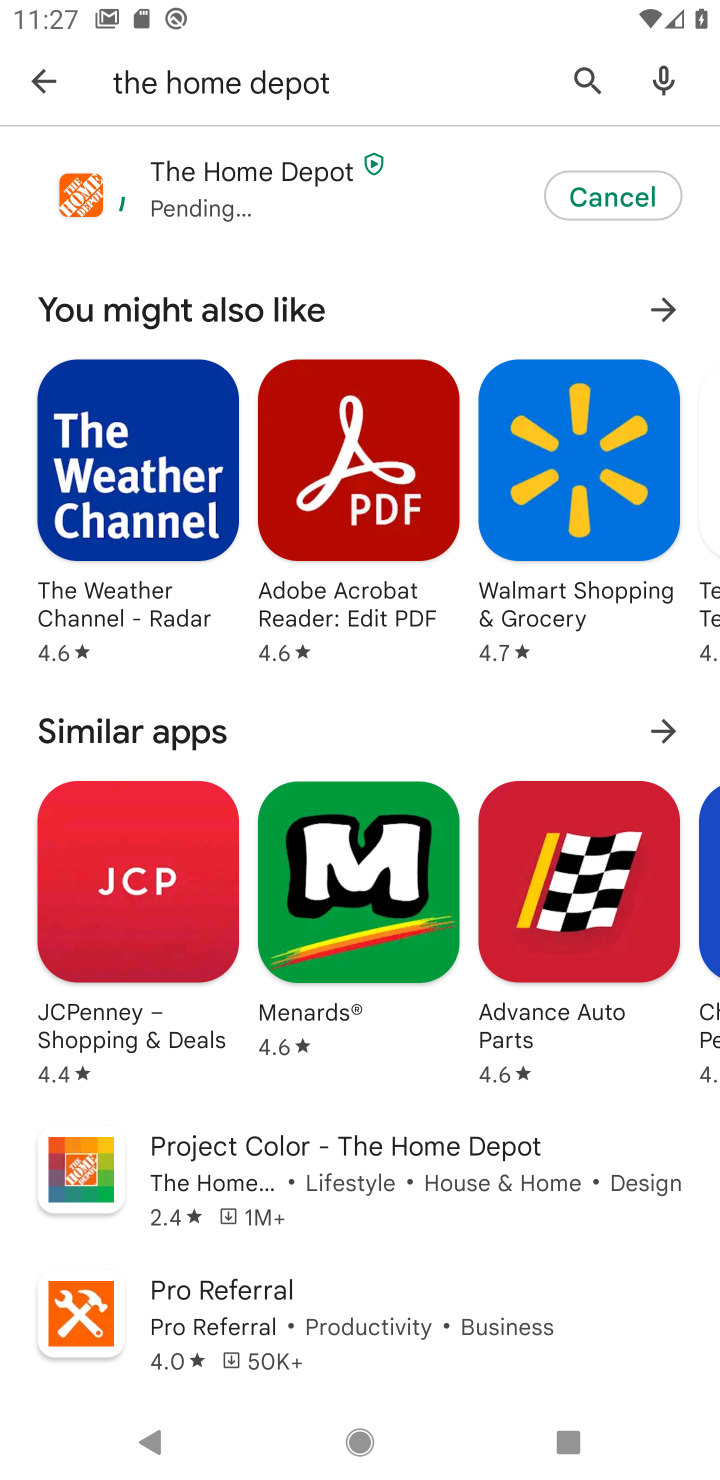
Step 63: click (620, 183)
Your task to perform on an android device: open app "The Home Depot" (install if not already installed) Image 64: 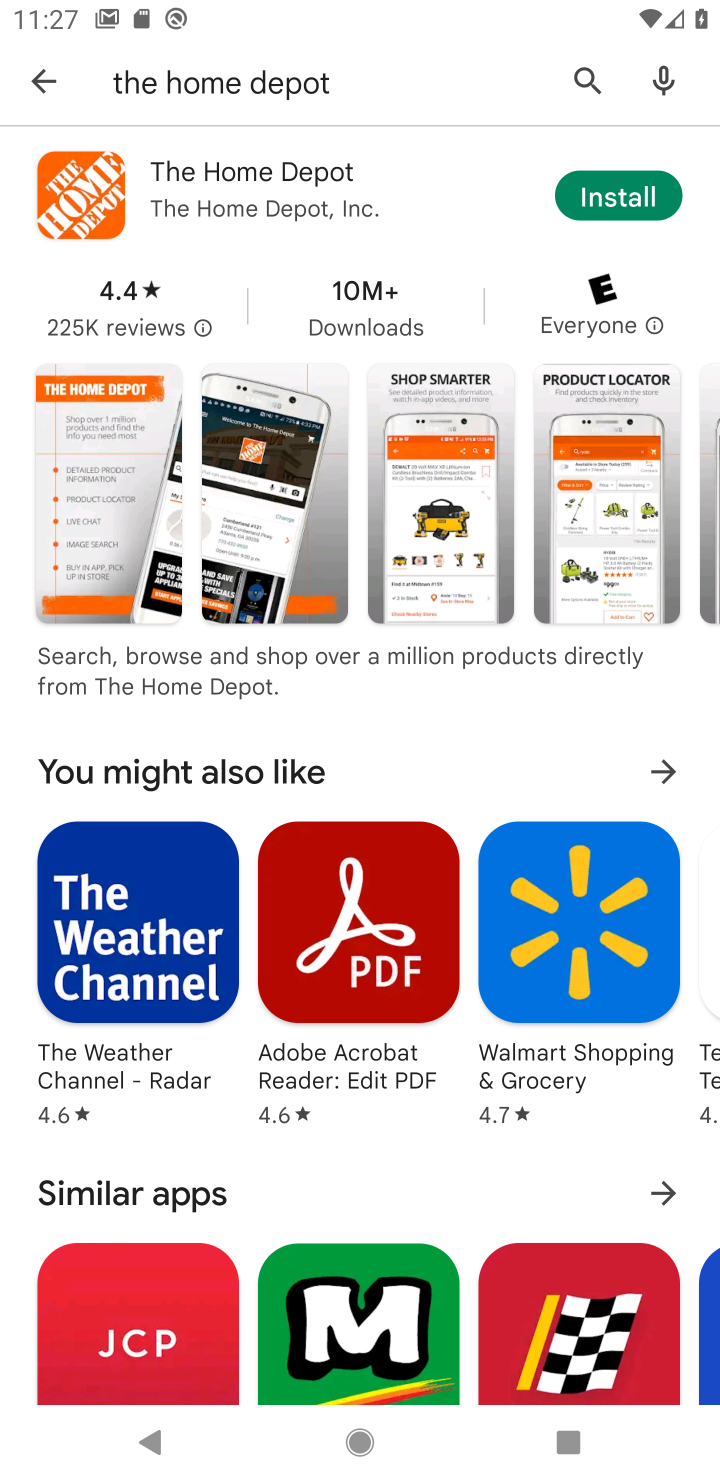
Step 64: click (648, 196)
Your task to perform on an android device: open app "The Home Depot" (install if not already installed) Image 65: 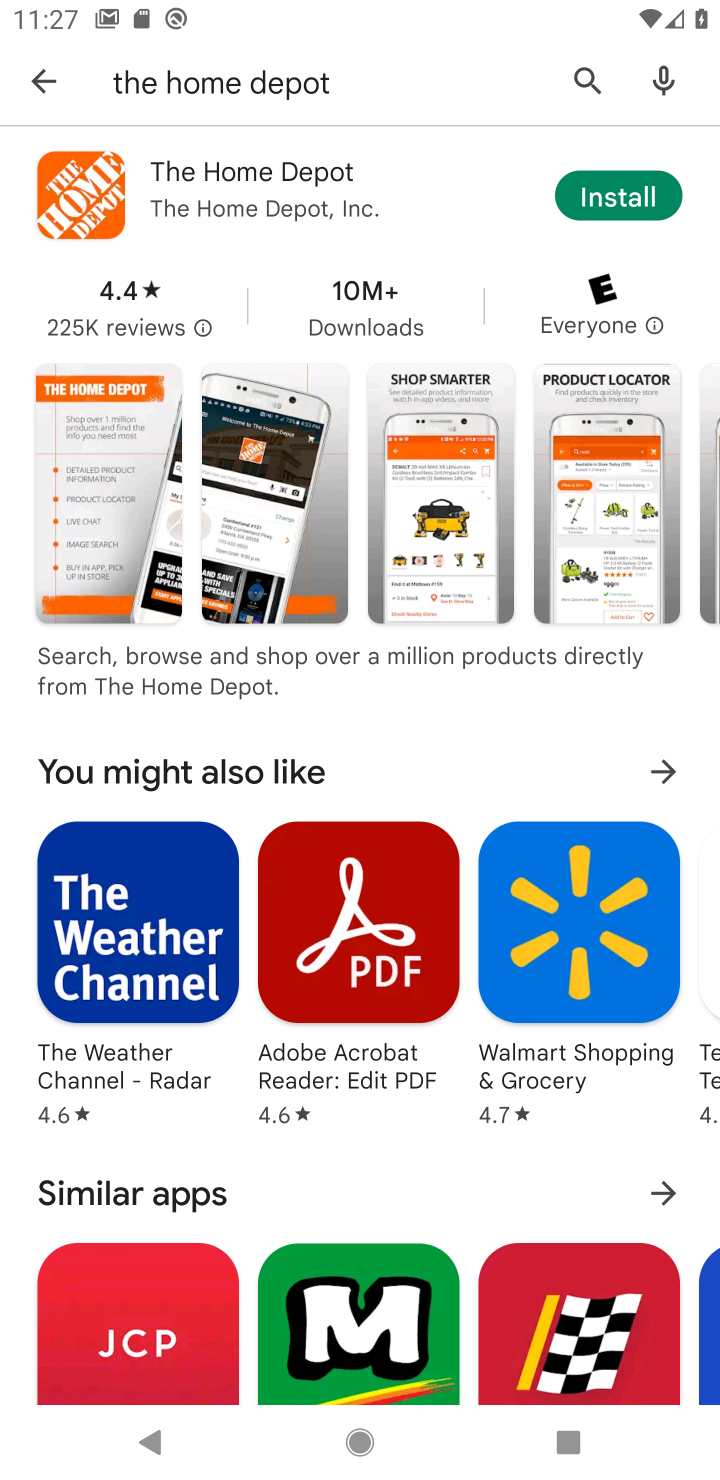
Step 65: click (648, 196)
Your task to perform on an android device: open app "The Home Depot" (install if not already installed) Image 66: 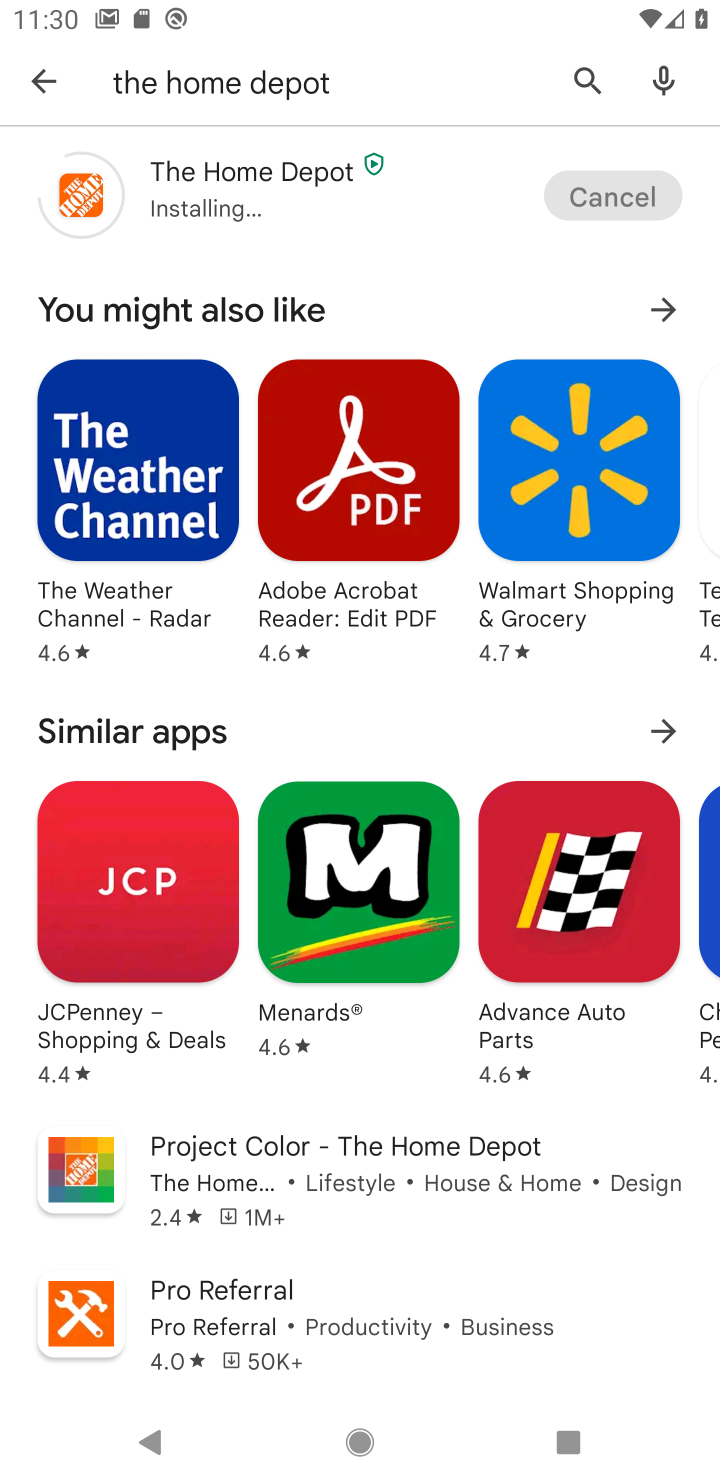
Step 66: task complete